Your task to perform on an android device: Open Google Chrome and click the shortcut for Amazon.com Image 0: 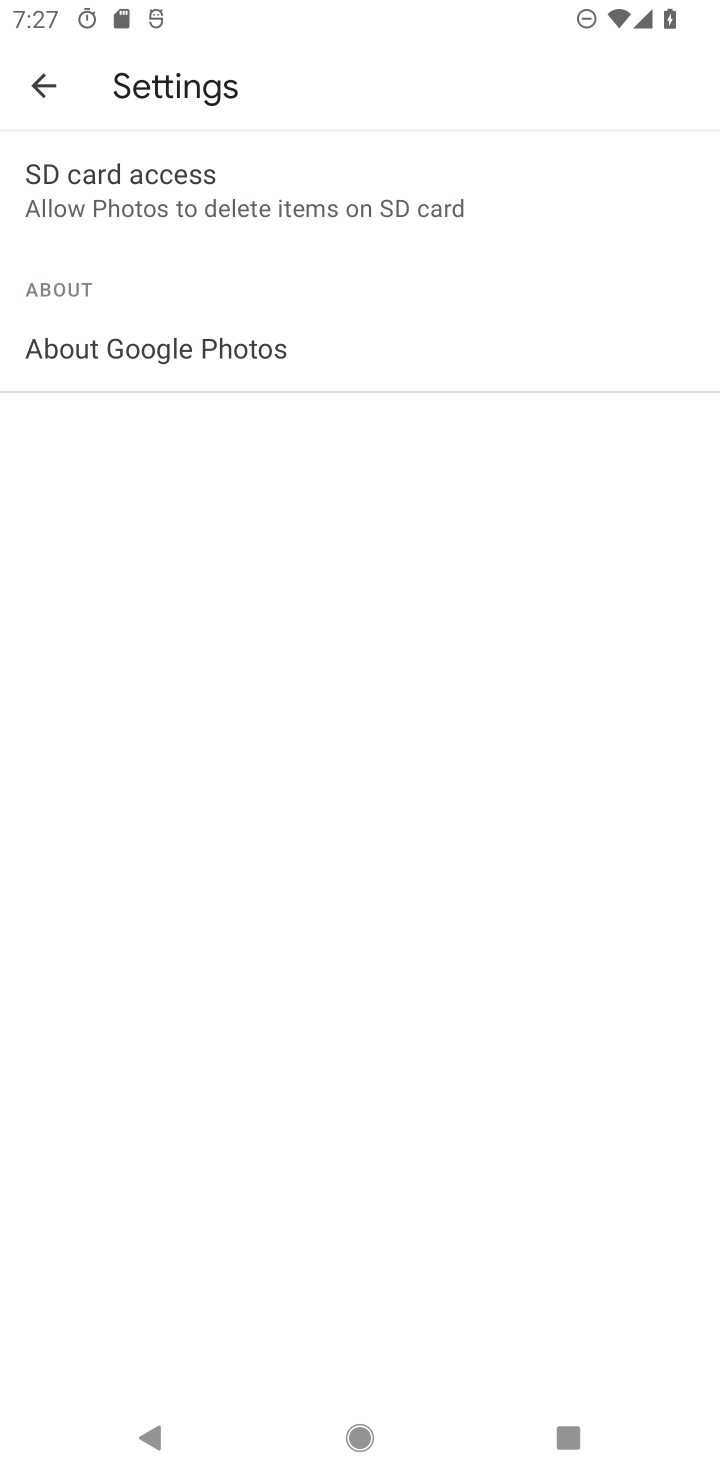
Step 0: press home button
Your task to perform on an android device: Open Google Chrome and click the shortcut for Amazon.com Image 1: 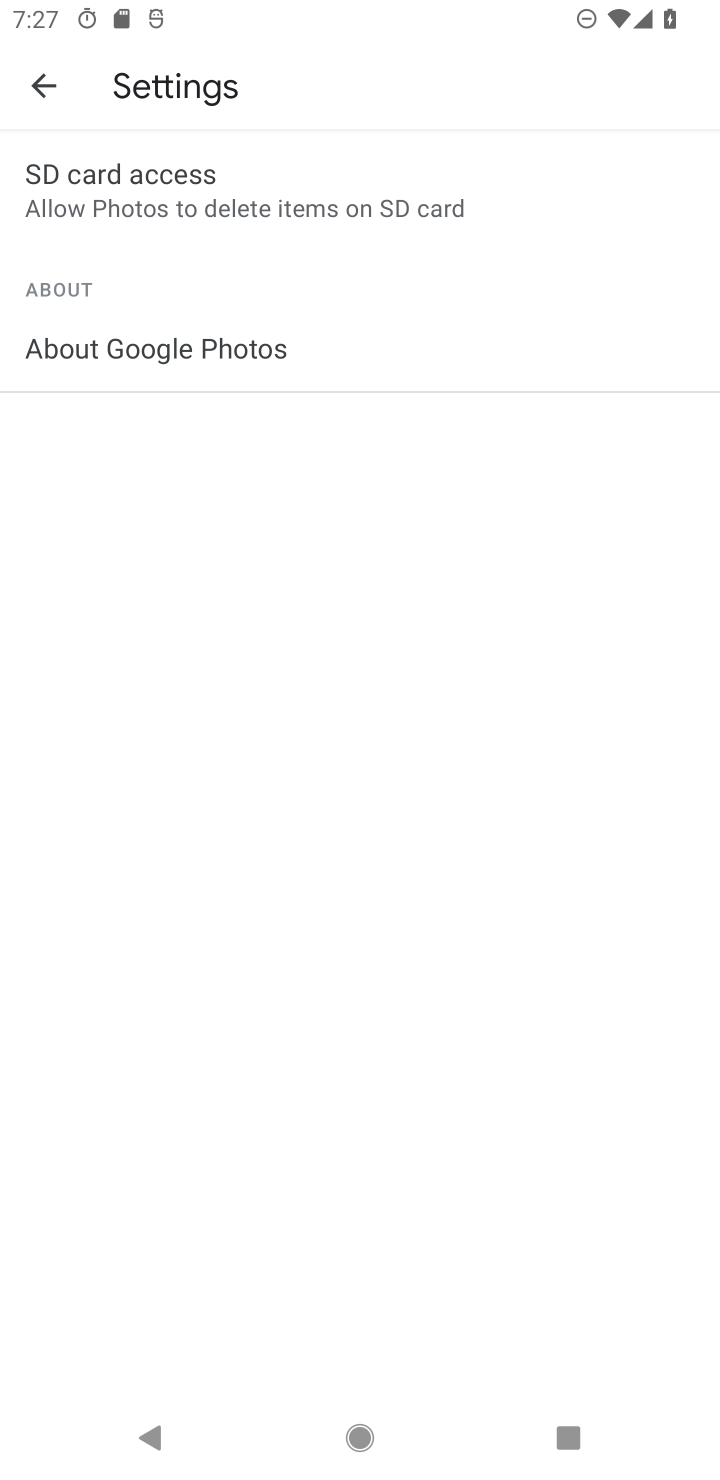
Step 1: drag from (459, 687) to (480, 224)
Your task to perform on an android device: Open Google Chrome and click the shortcut for Amazon.com Image 2: 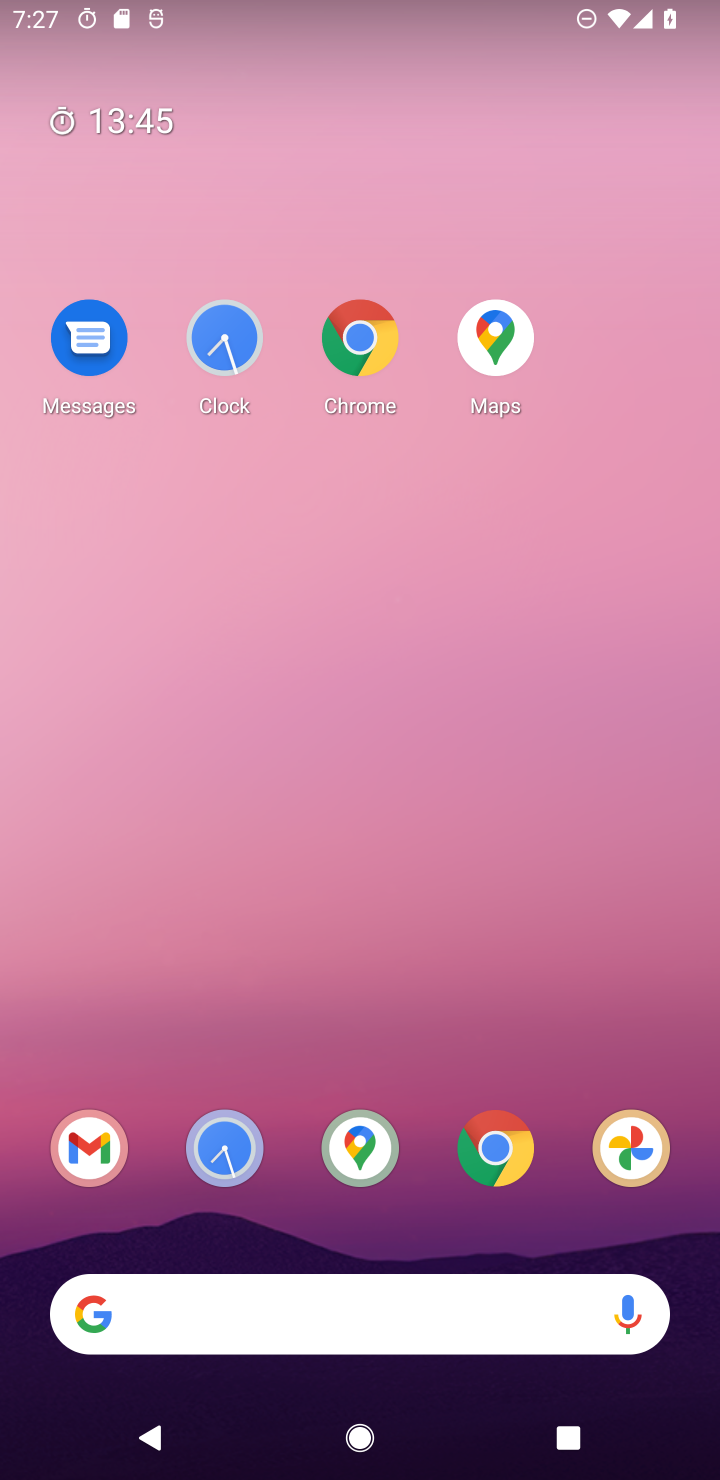
Step 2: drag from (416, 1092) to (445, 138)
Your task to perform on an android device: Open Google Chrome and click the shortcut for Amazon.com Image 3: 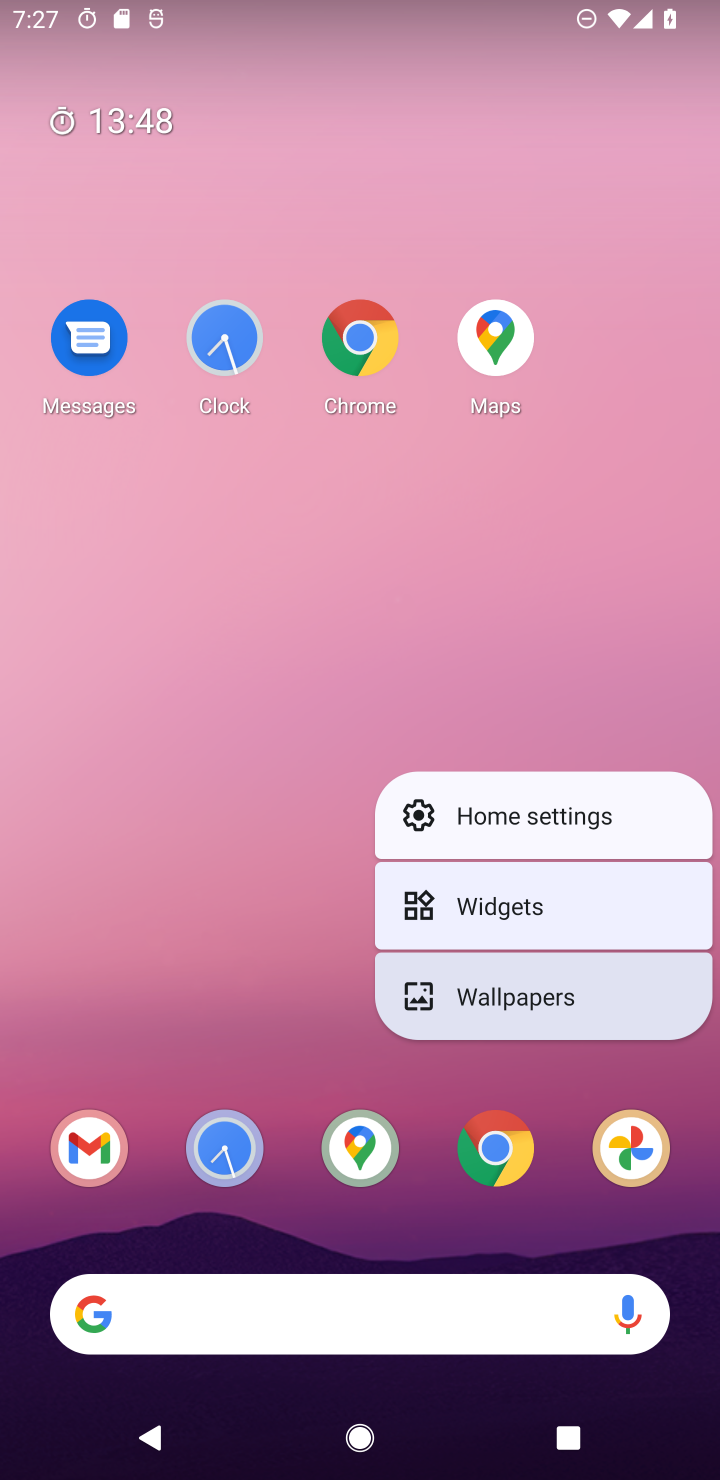
Step 3: click (498, 1144)
Your task to perform on an android device: Open Google Chrome and click the shortcut for Amazon.com Image 4: 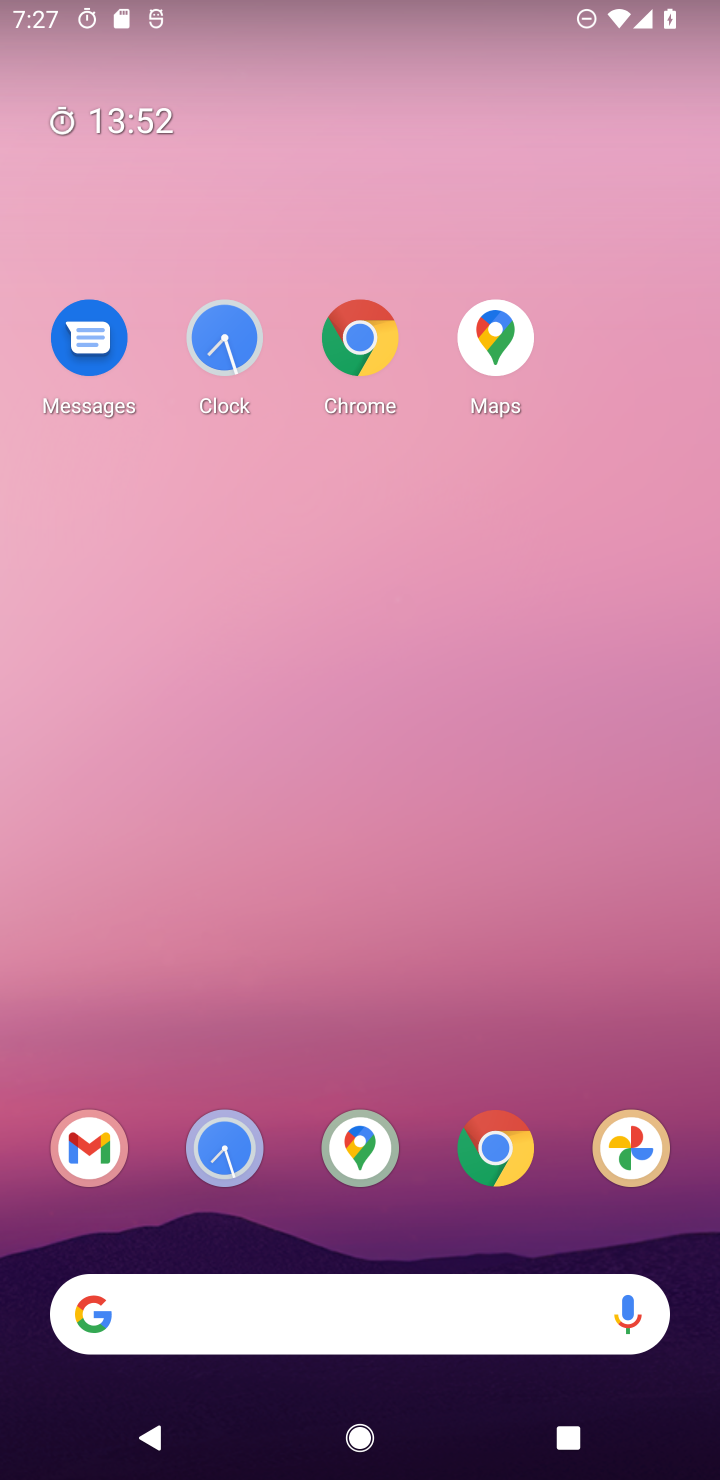
Step 4: click (488, 1131)
Your task to perform on an android device: Open Google Chrome and click the shortcut for Amazon.com Image 5: 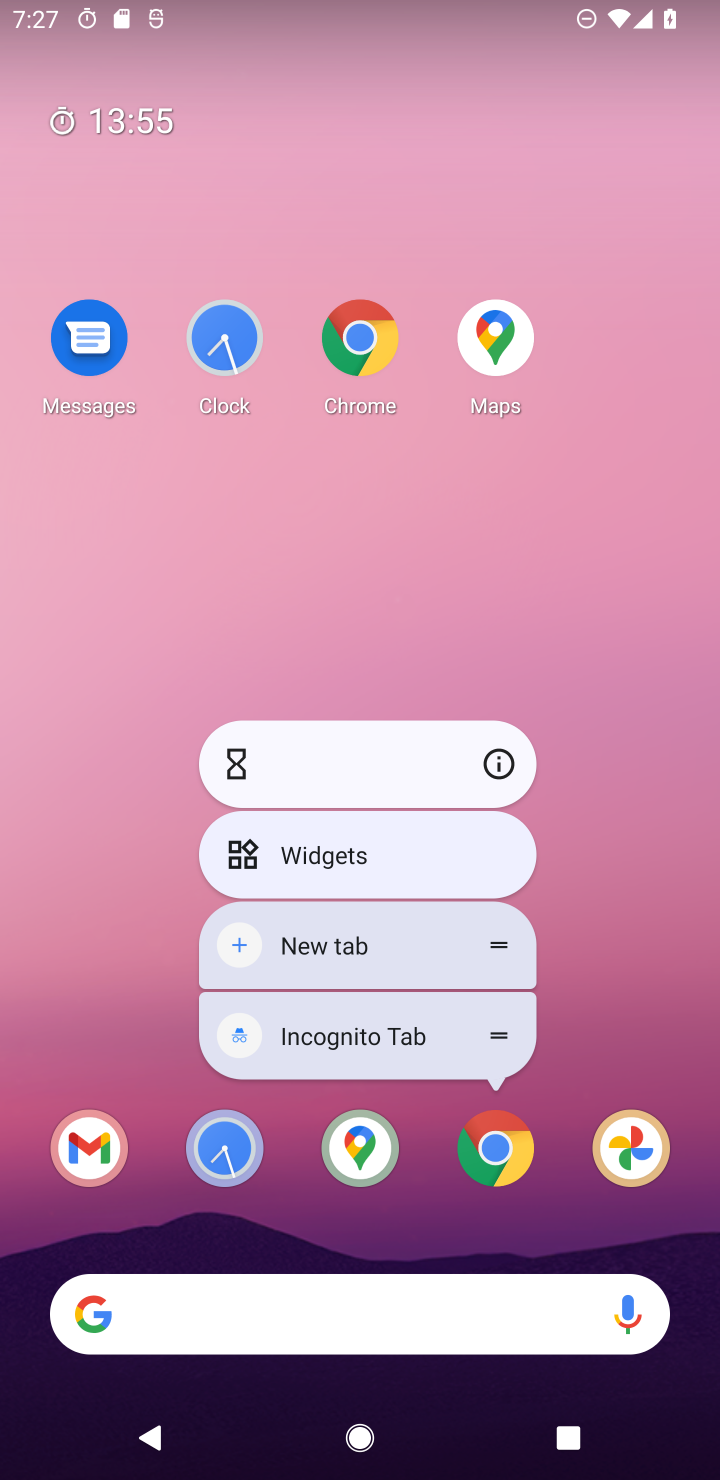
Step 5: click (482, 742)
Your task to perform on an android device: Open Google Chrome and click the shortcut for Amazon.com Image 6: 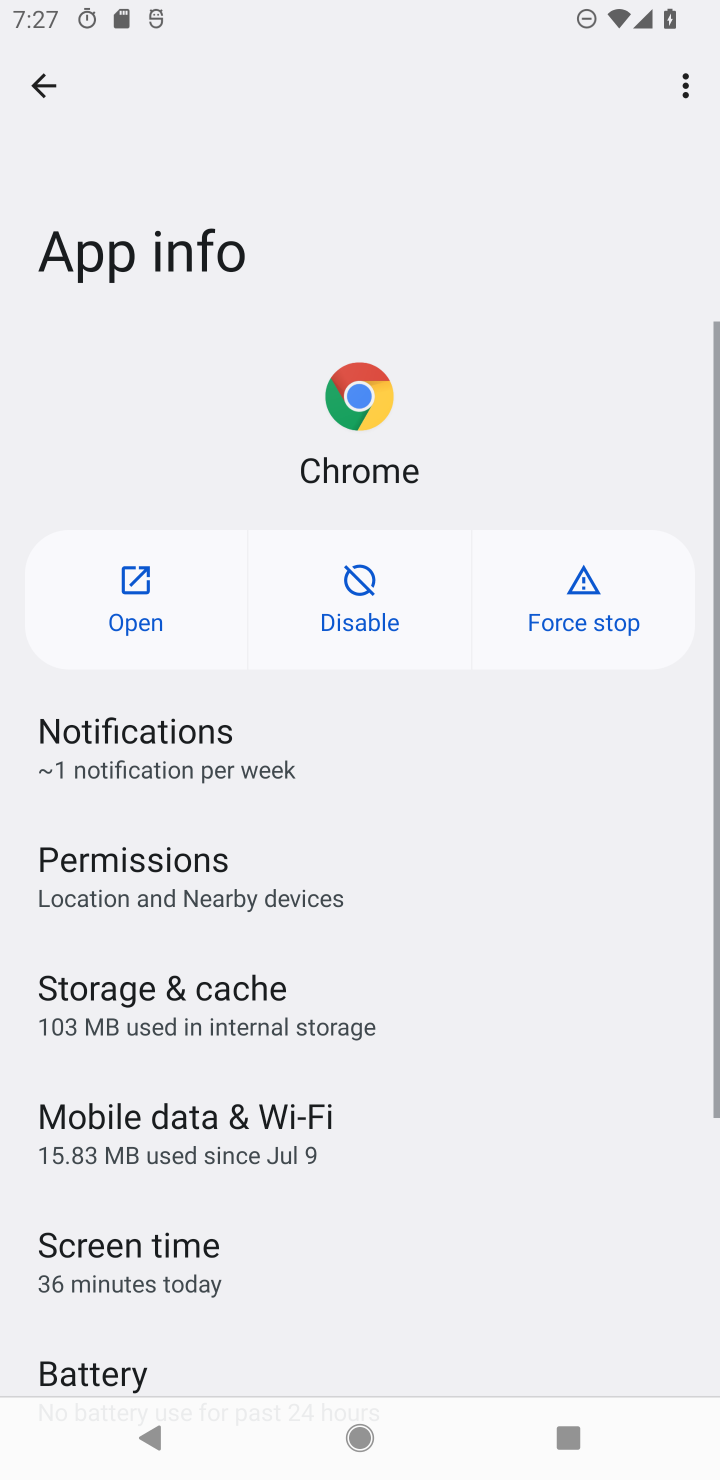
Step 6: click (137, 569)
Your task to perform on an android device: Open Google Chrome and click the shortcut for Amazon.com Image 7: 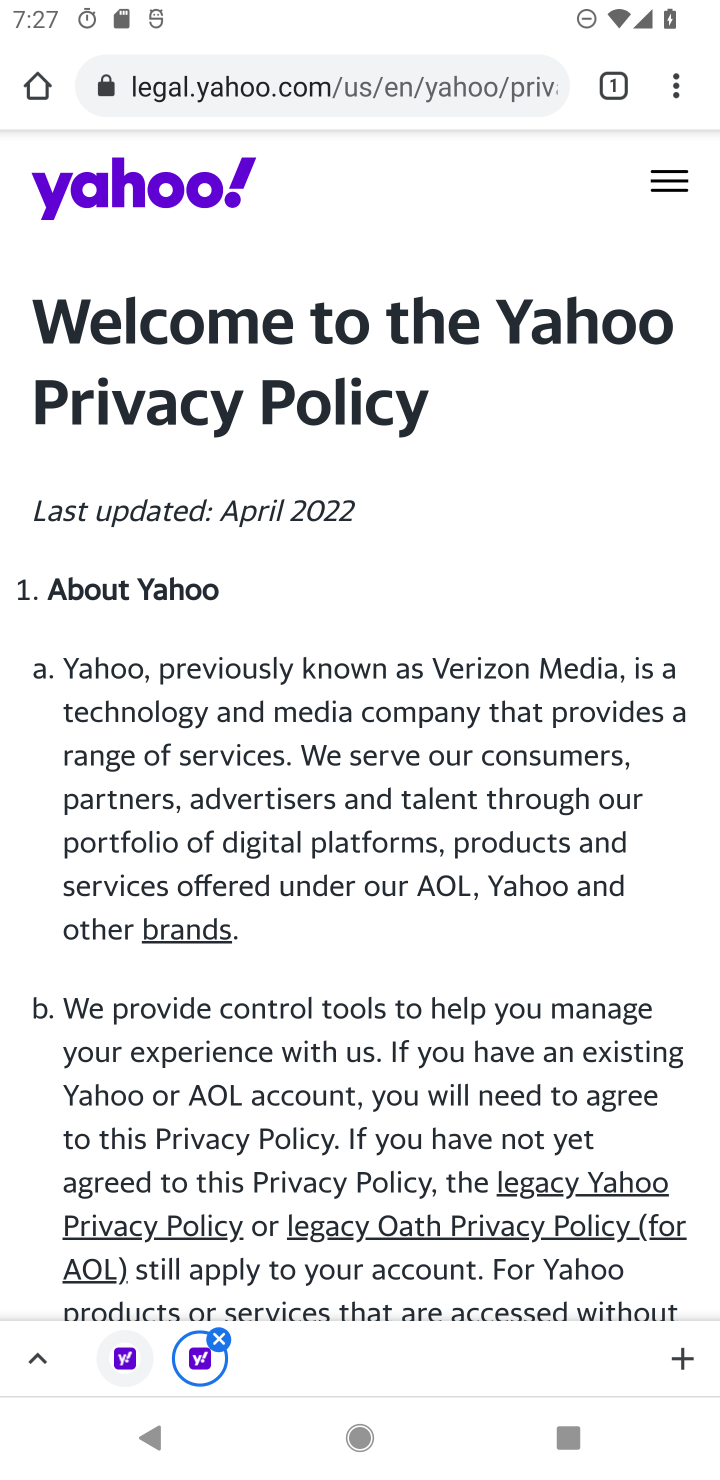
Step 7: click (620, 89)
Your task to perform on an android device: Open Google Chrome and click the shortcut for Amazon.com Image 8: 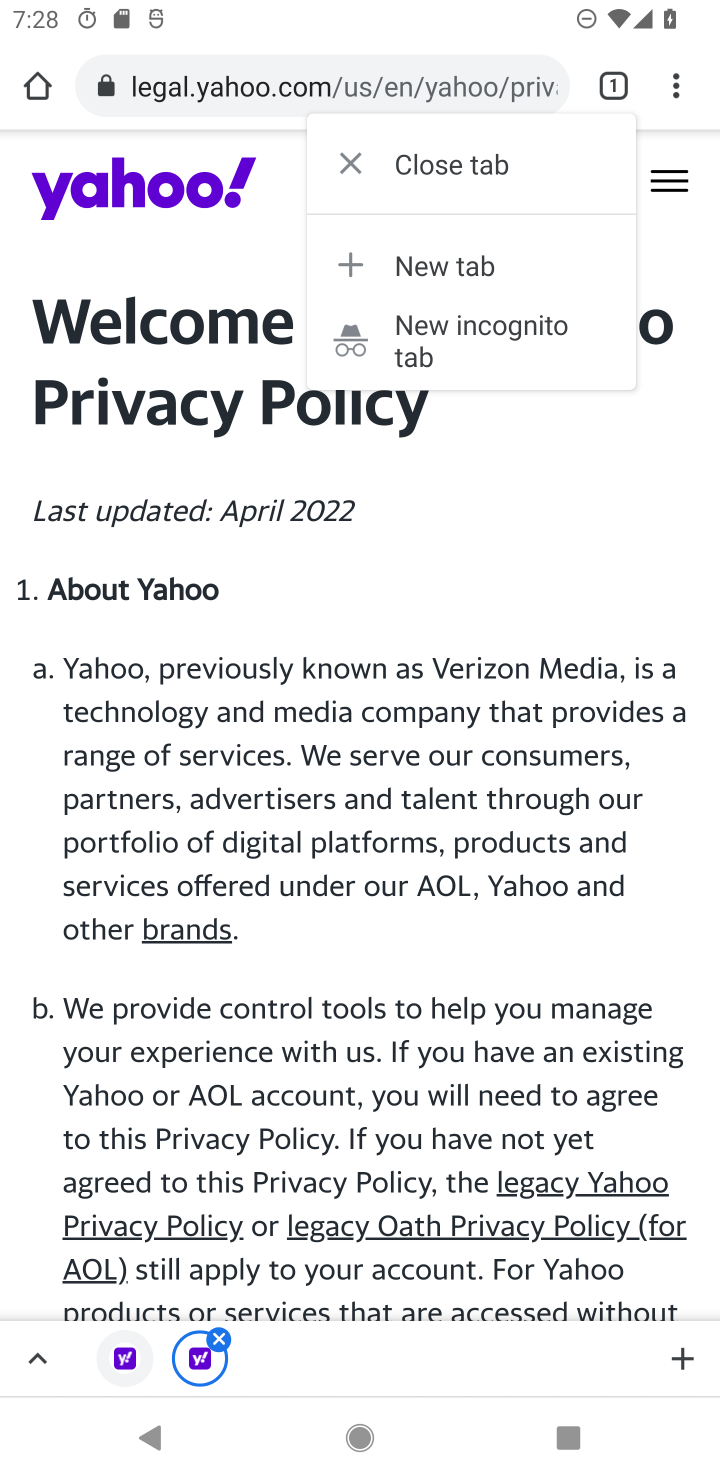
Step 8: click (492, 264)
Your task to perform on an android device: Open Google Chrome and click the shortcut for Amazon.com Image 9: 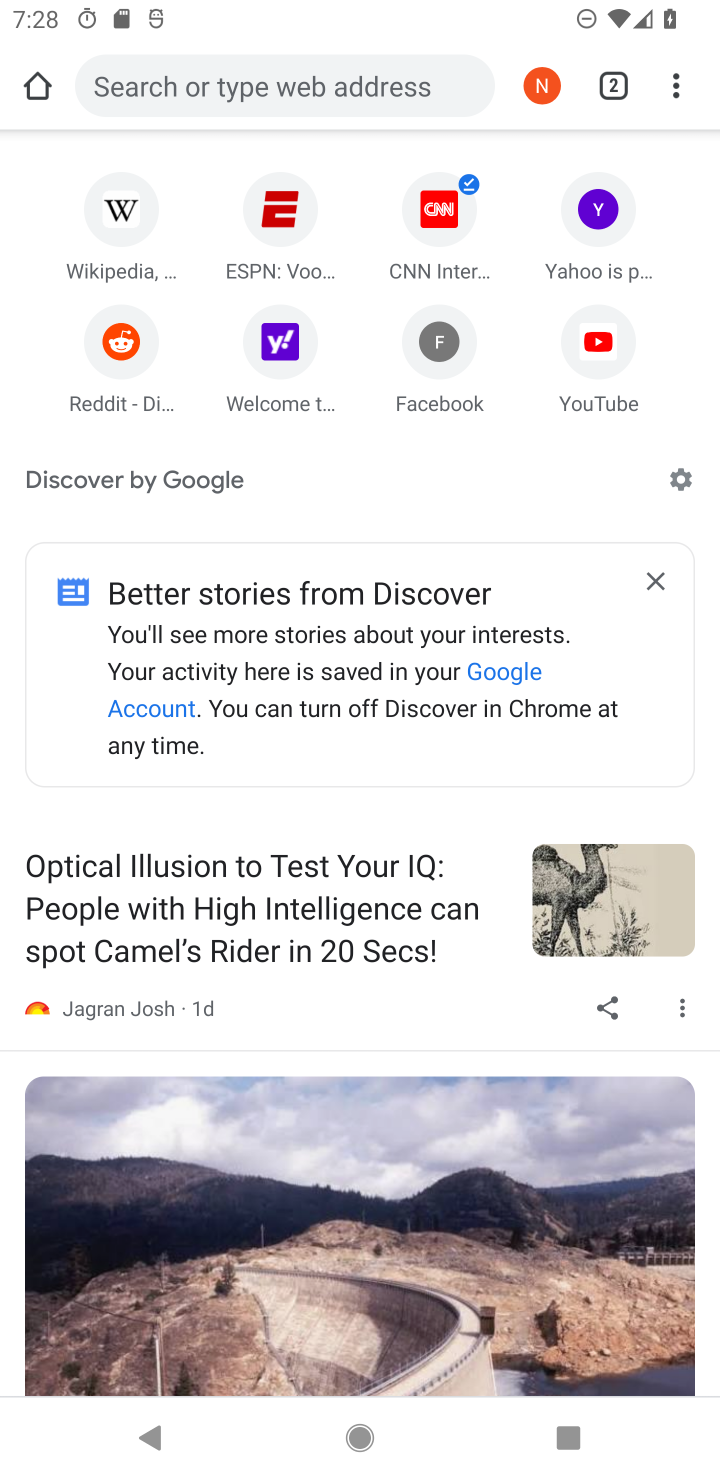
Step 9: drag from (380, 905) to (386, 260)
Your task to perform on an android device: Open Google Chrome and click the shortcut for Amazon.com Image 10: 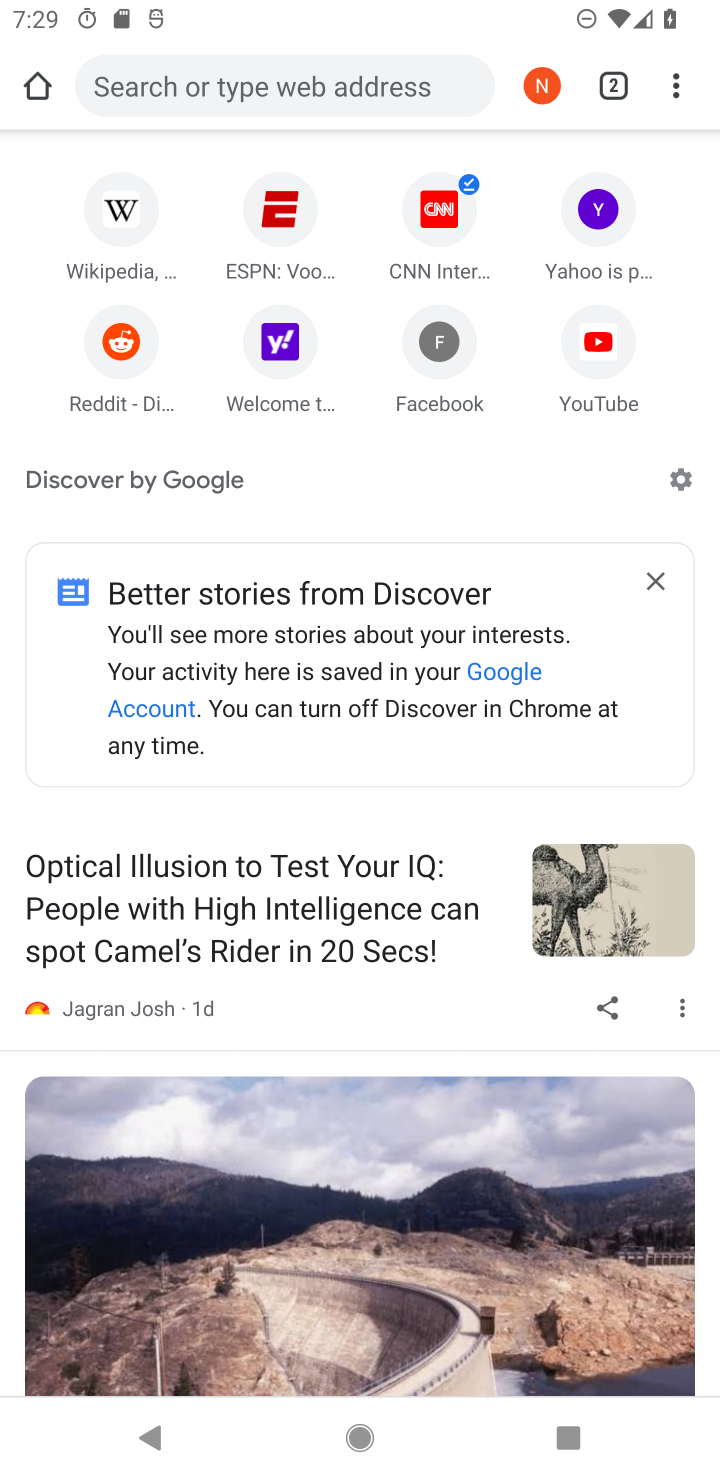
Step 10: drag from (377, 698) to (411, 337)
Your task to perform on an android device: Open Google Chrome and click the shortcut for Amazon.com Image 11: 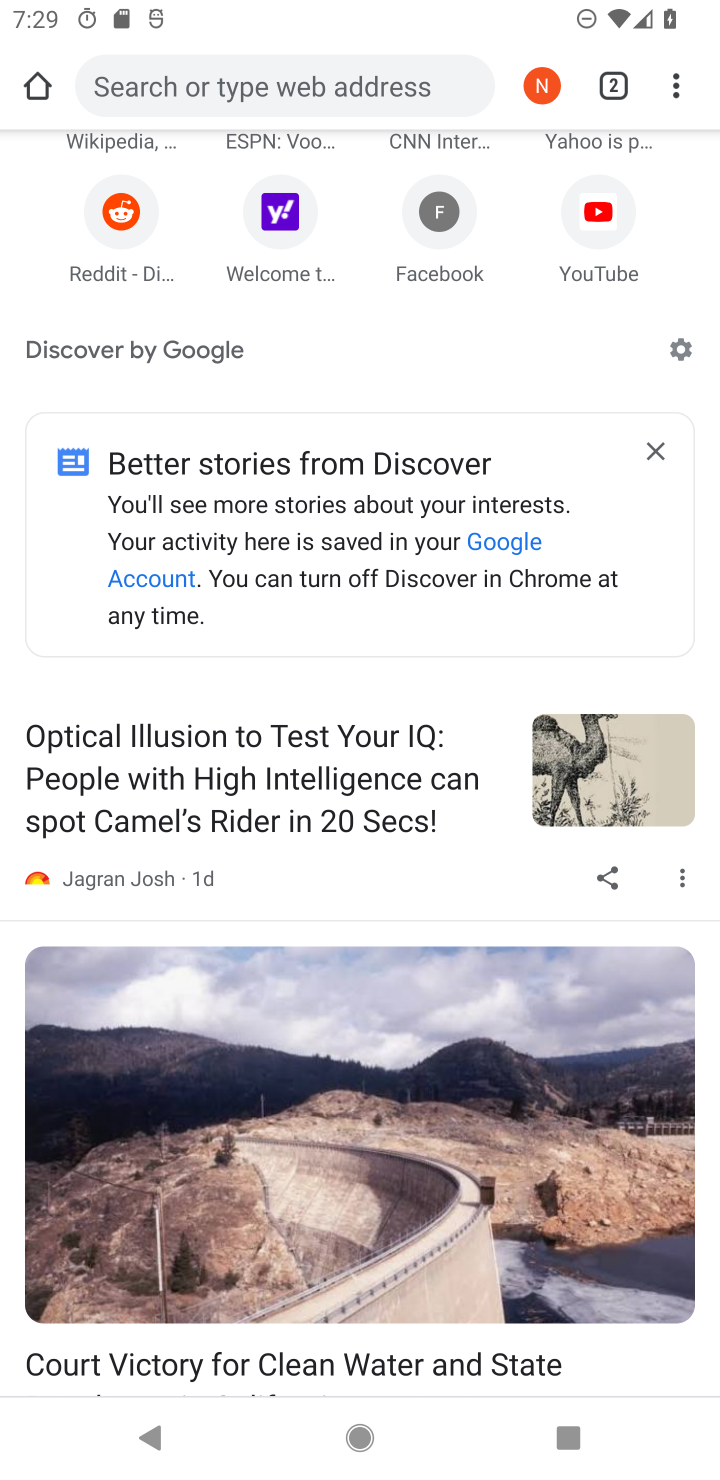
Step 11: drag from (442, 434) to (442, 265)
Your task to perform on an android device: Open Google Chrome and click the shortcut for Amazon.com Image 12: 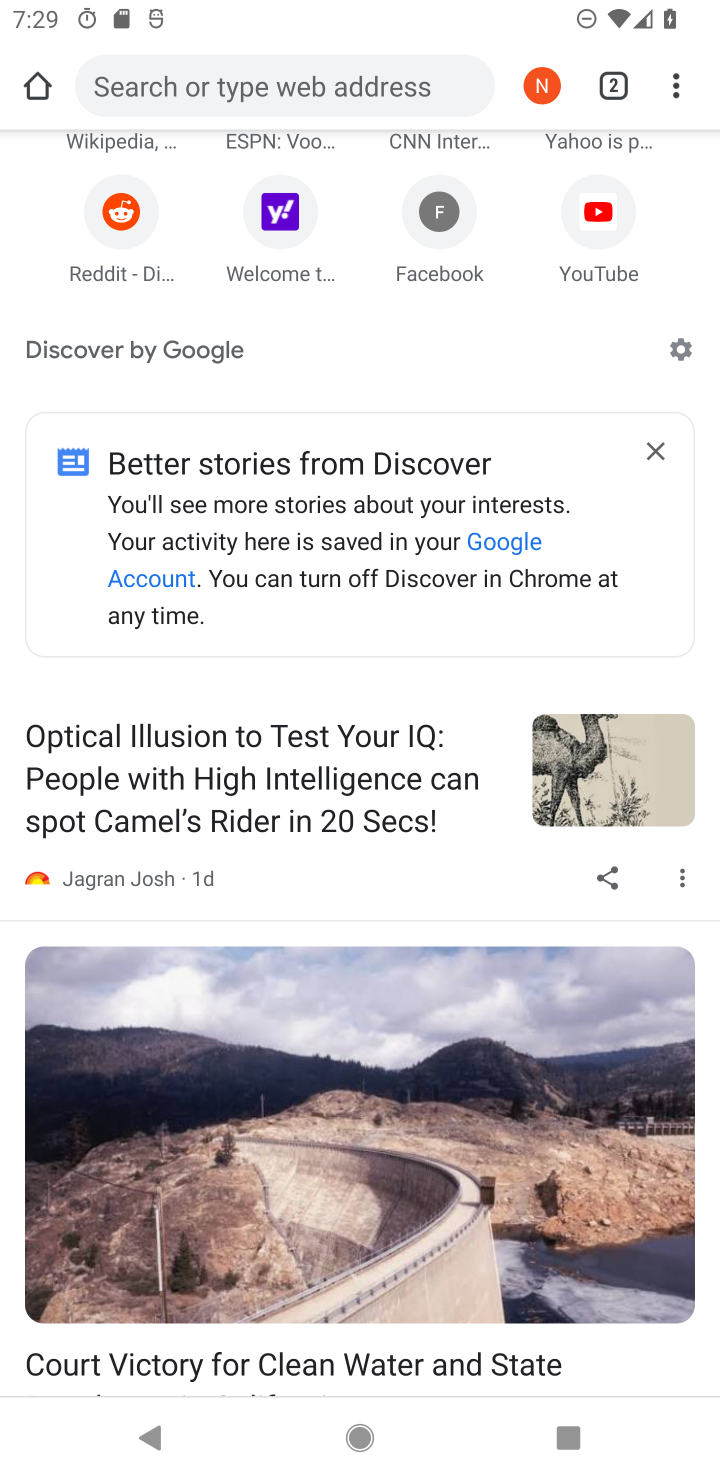
Step 12: drag from (376, 741) to (376, 358)
Your task to perform on an android device: Open Google Chrome and click the shortcut for Amazon.com Image 13: 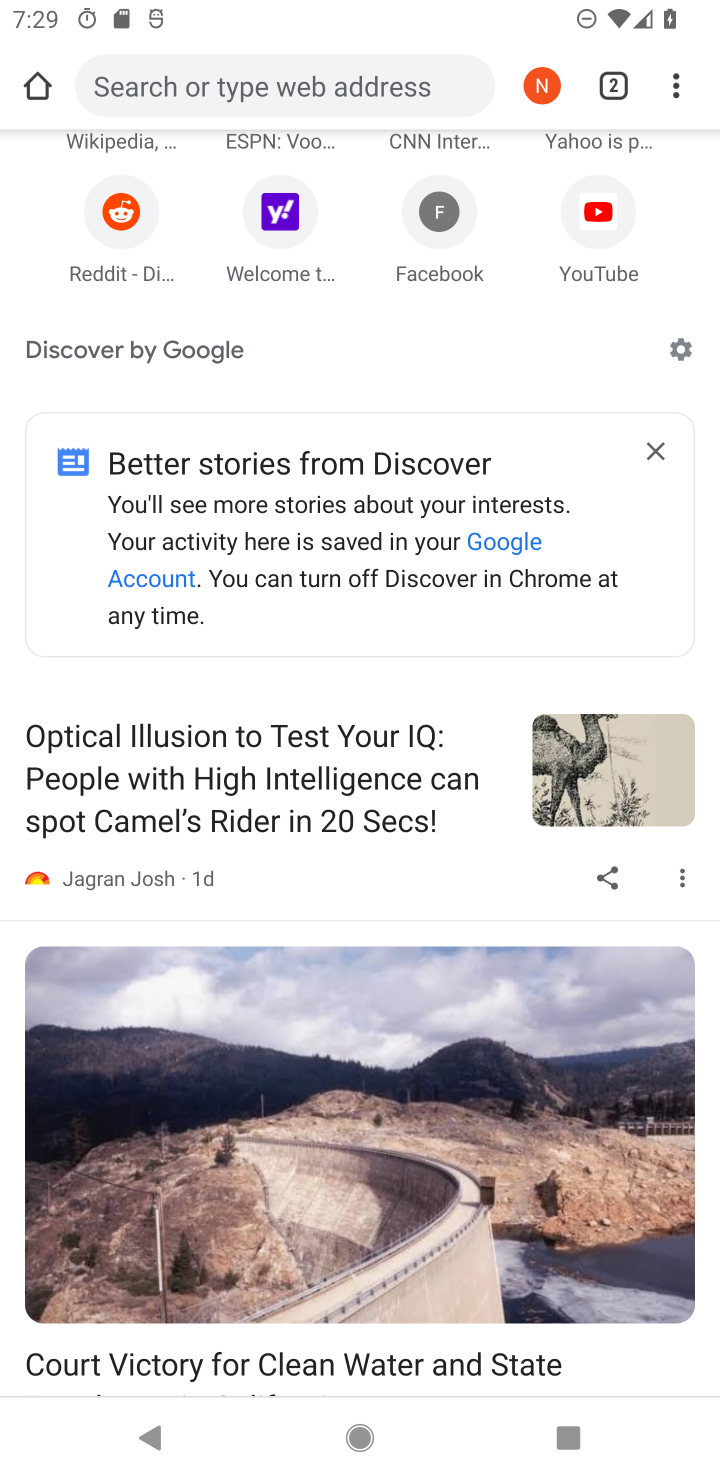
Step 13: click (557, 1449)
Your task to perform on an android device: Open Google Chrome and click the shortcut for Amazon.com Image 14: 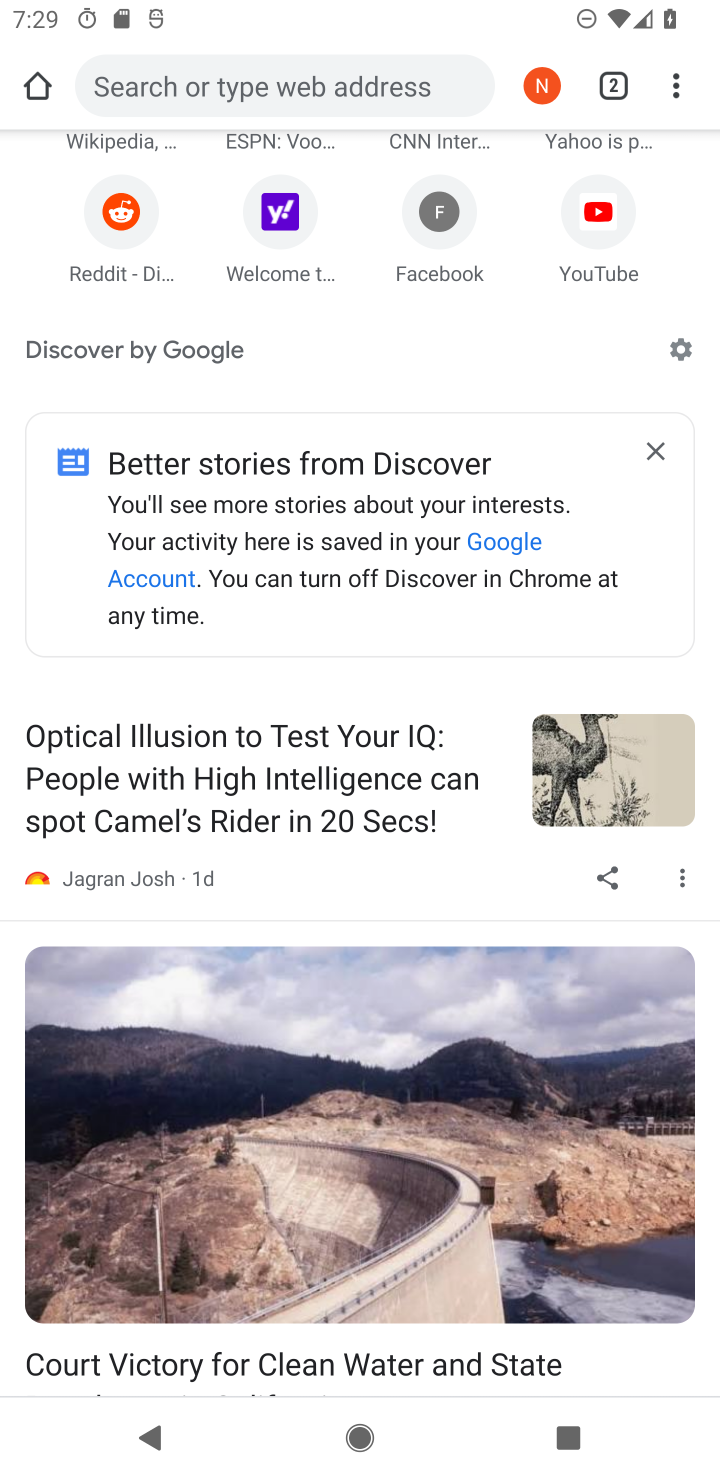
Step 14: click (171, 90)
Your task to perform on an android device: Open Google Chrome and click the shortcut for Amazon.com Image 15: 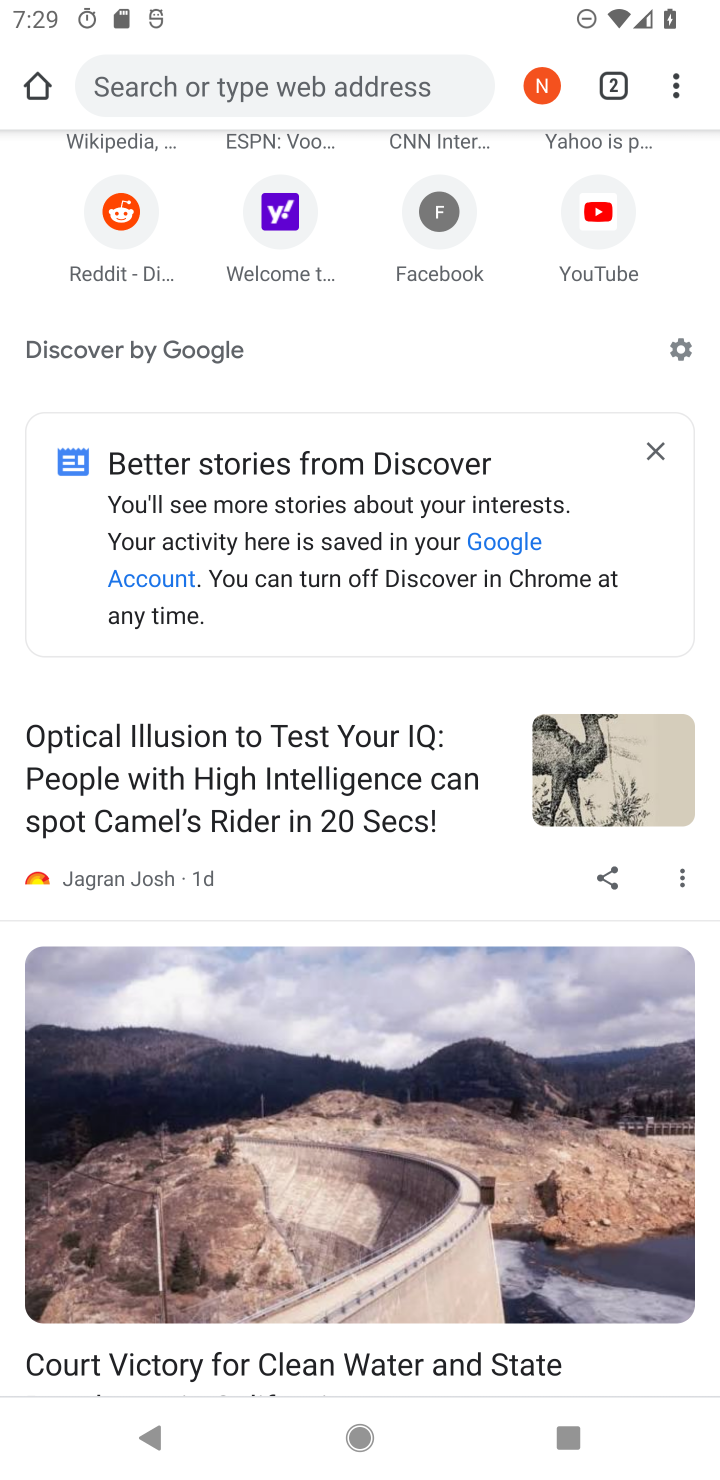
Step 15: drag from (415, 727) to (516, 1286)
Your task to perform on an android device: Open Google Chrome and click the shortcut for Amazon.com Image 16: 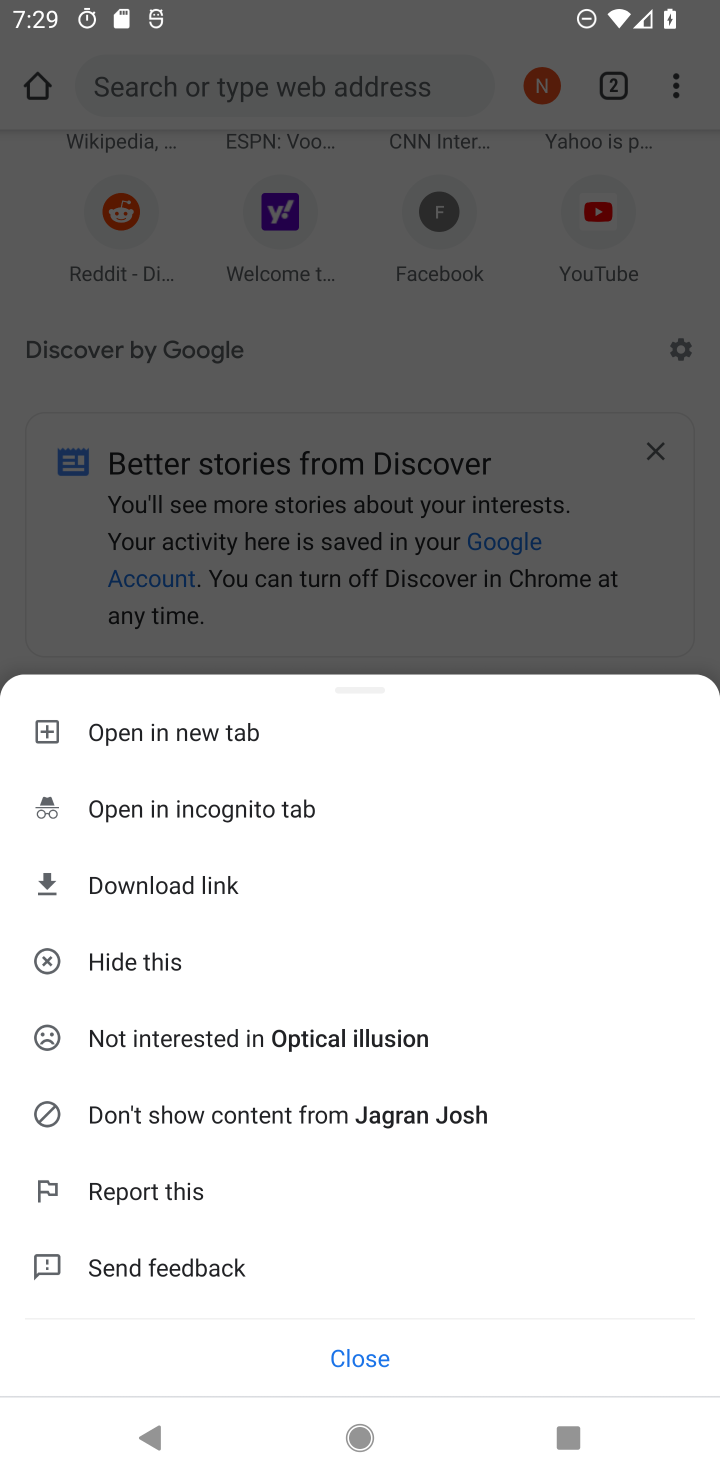
Step 16: drag from (378, 425) to (305, 1254)
Your task to perform on an android device: Open Google Chrome and click the shortcut for Amazon.com Image 17: 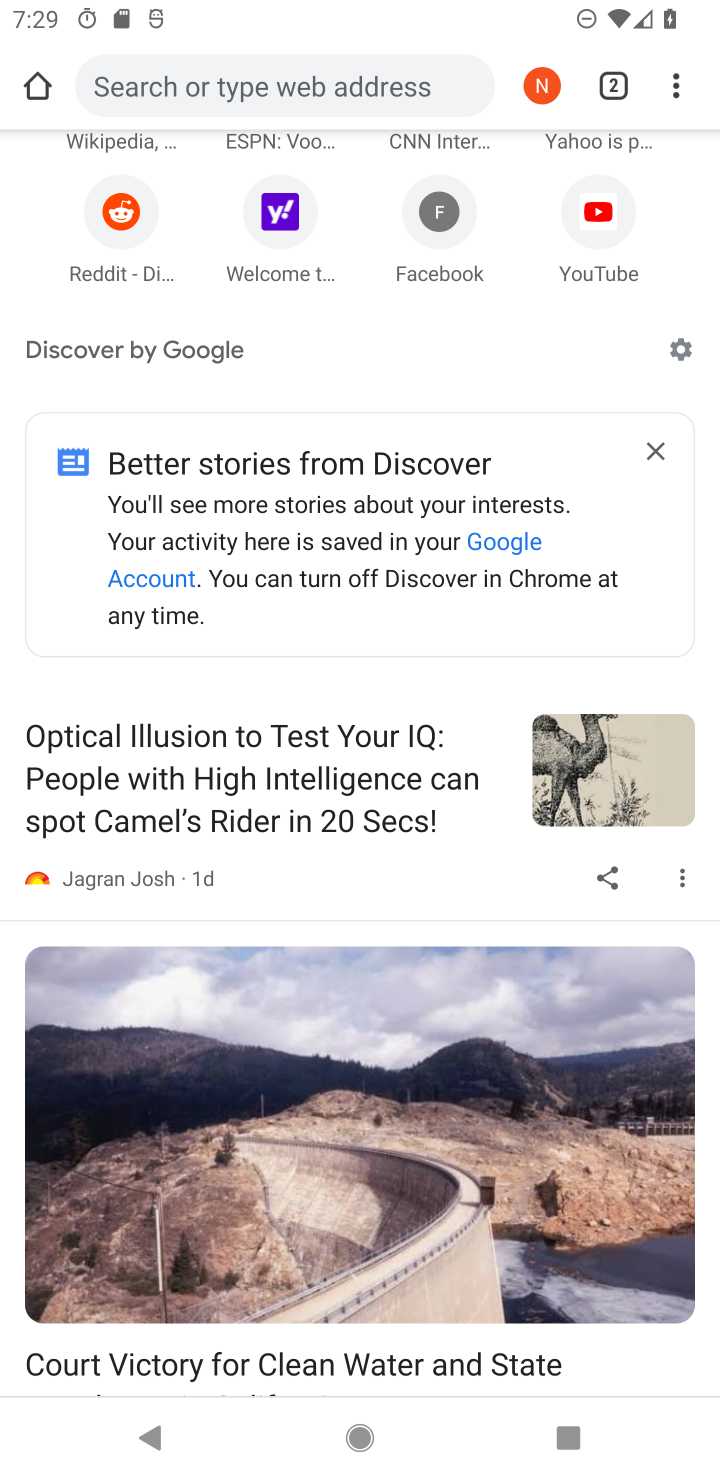
Step 17: click (350, 1365)
Your task to perform on an android device: Open Google Chrome and click the shortcut for Amazon.com Image 18: 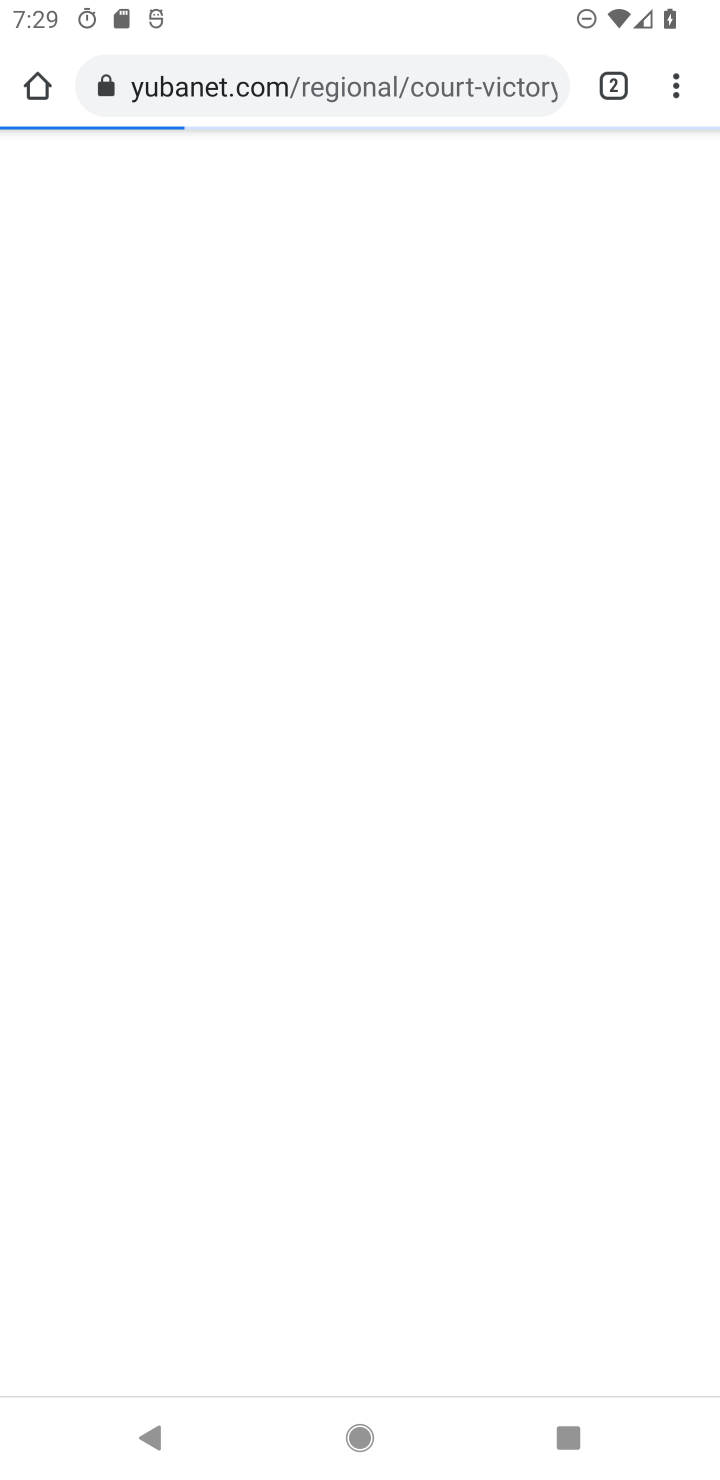
Step 18: drag from (452, 1139) to (551, 1445)
Your task to perform on an android device: Open Google Chrome and click the shortcut for Amazon.com Image 19: 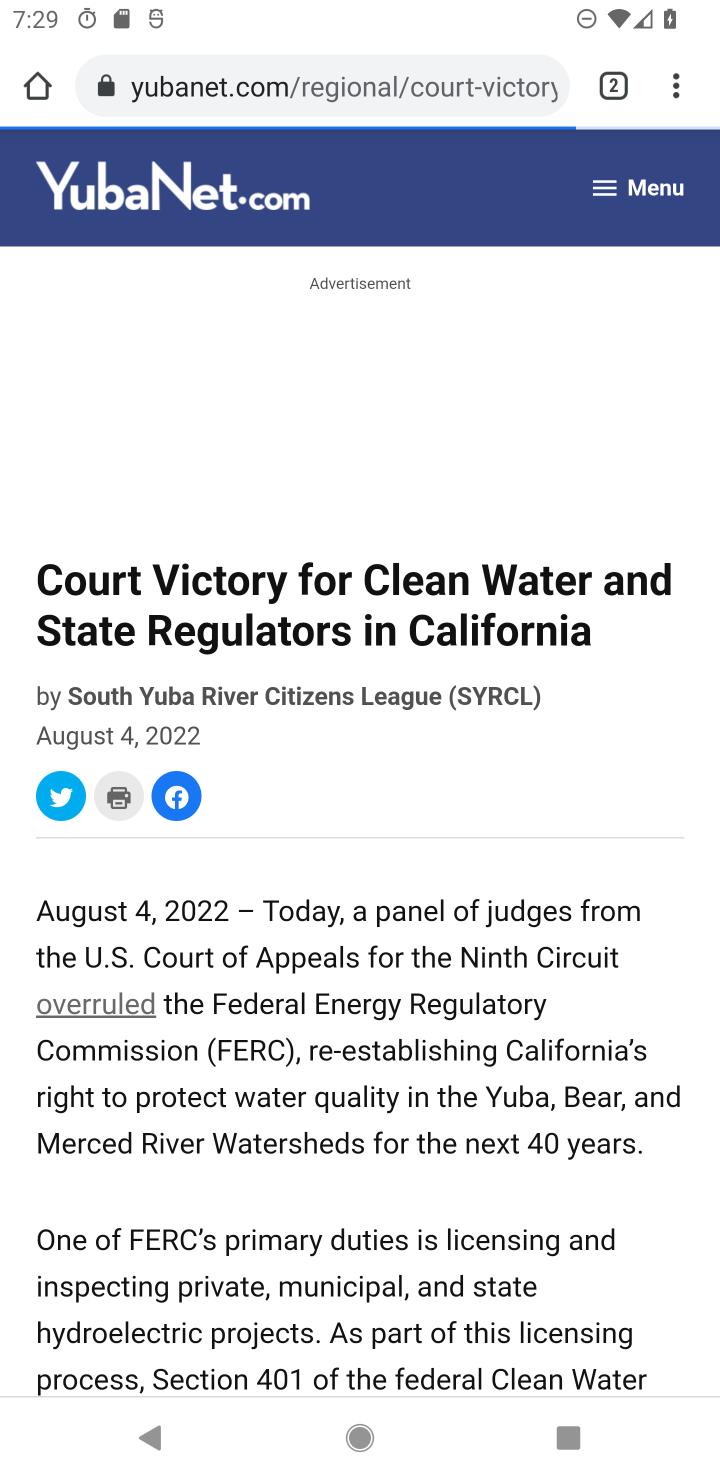
Step 19: drag from (332, 327) to (487, 1135)
Your task to perform on an android device: Open Google Chrome and click the shortcut for Amazon.com Image 20: 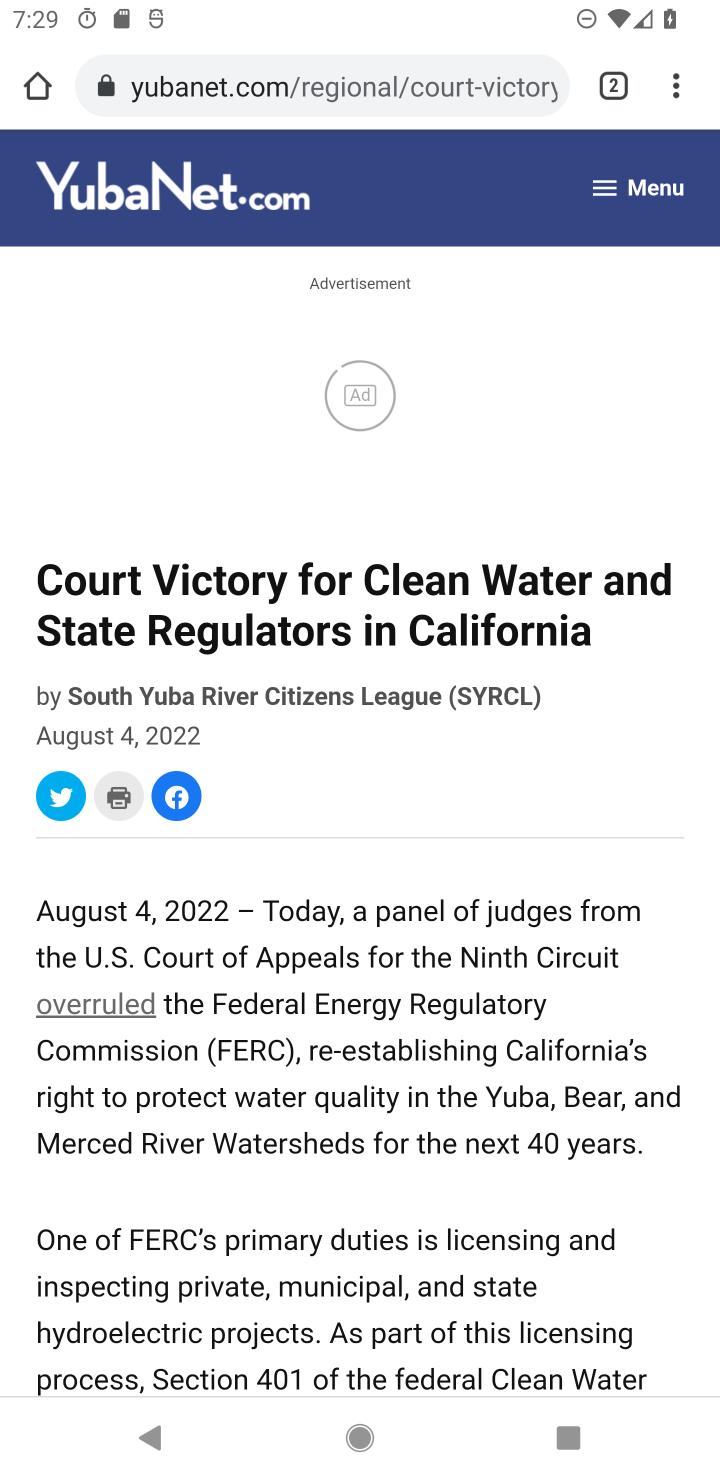
Step 20: click (262, 94)
Your task to perform on an android device: Open Google Chrome and click the shortcut for Amazon.com Image 21: 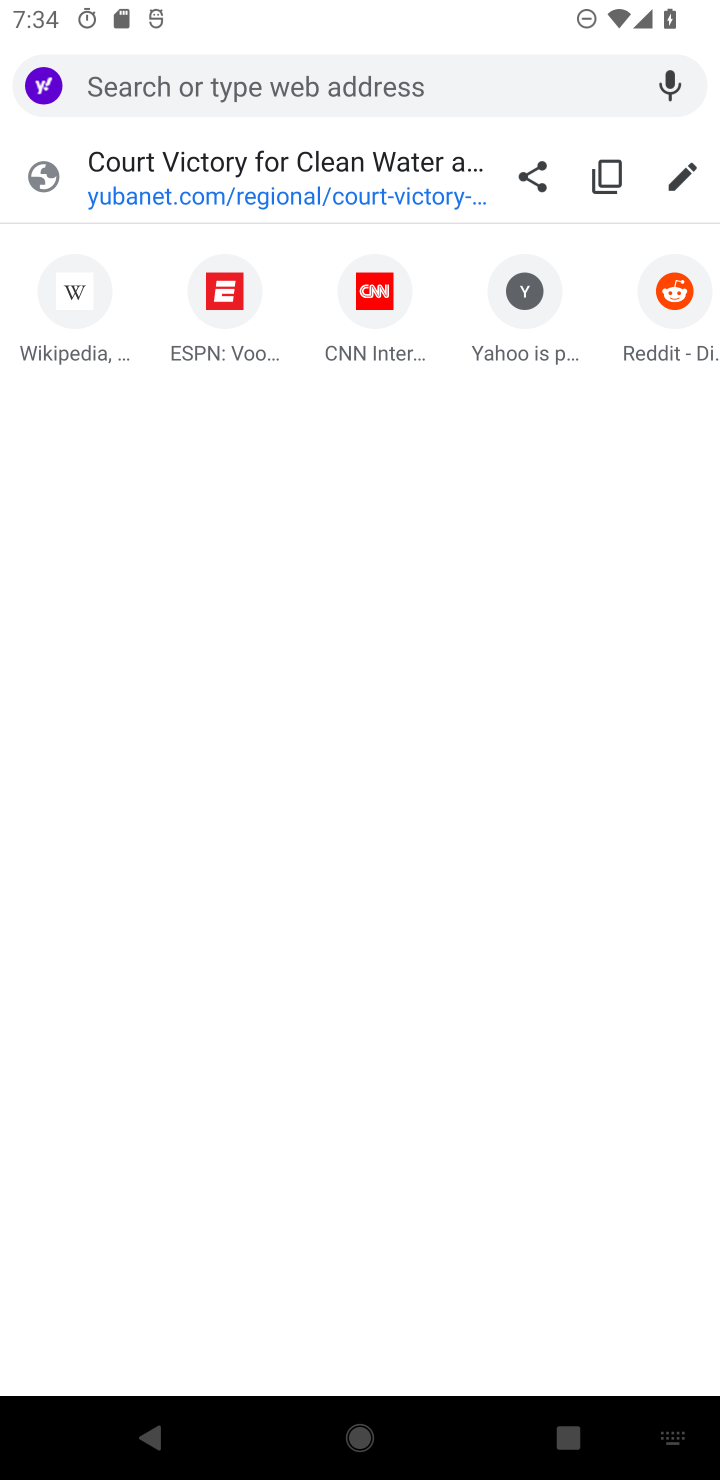
Step 21: click (392, 604)
Your task to perform on an android device: Open Google Chrome and click the shortcut for Amazon.com Image 22: 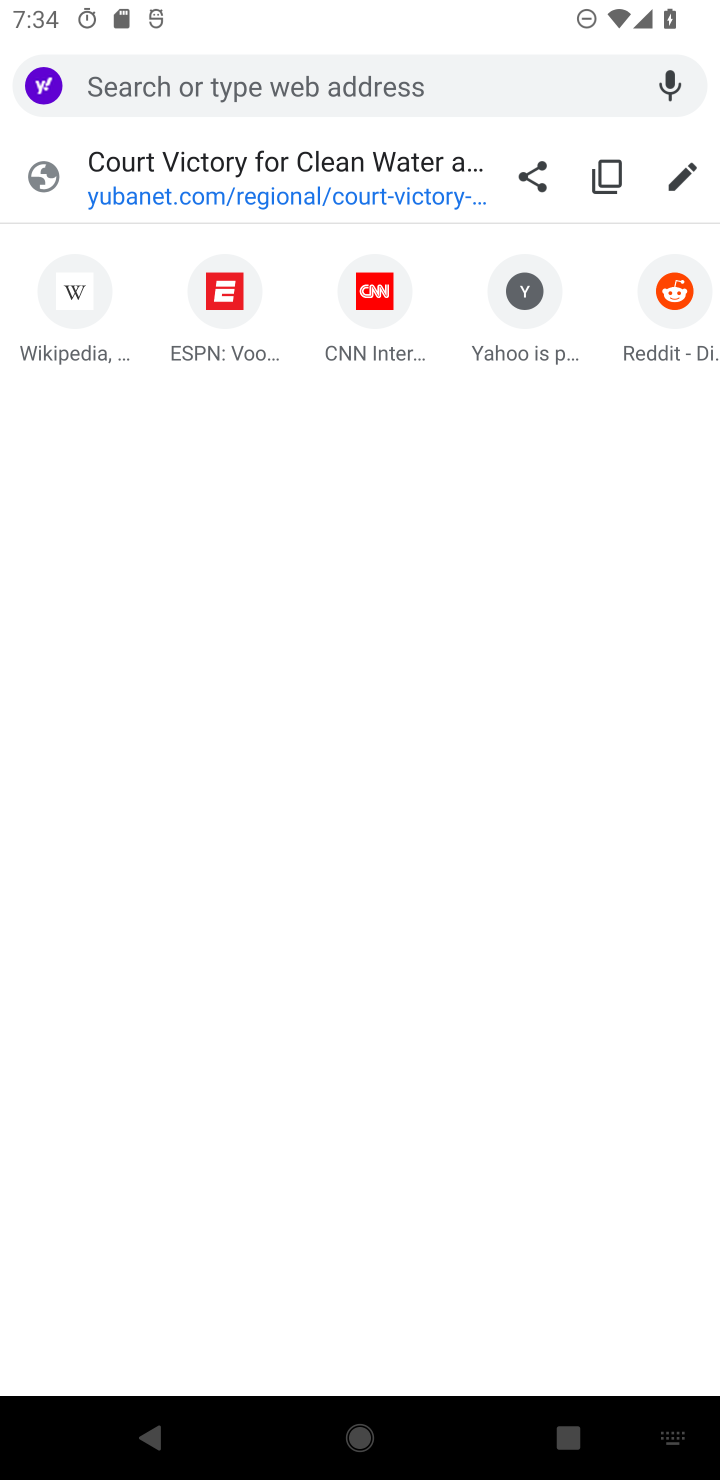
Step 22: click (391, 922)
Your task to perform on an android device: Open Google Chrome and click the shortcut for Amazon.com Image 23: 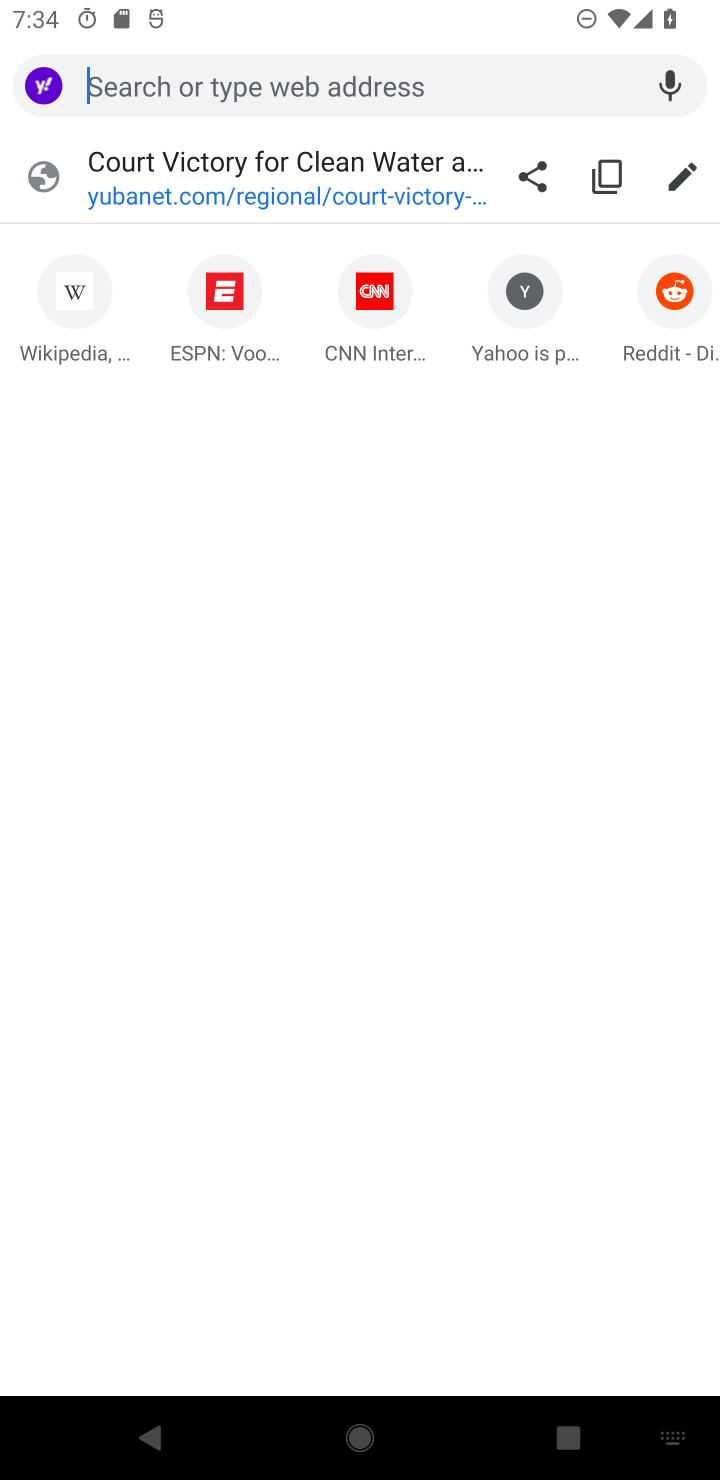
Step 23: press home button
Your task to perform on an android device: Open Google Chrome and click the shortcut for Amazon.com Image 24: 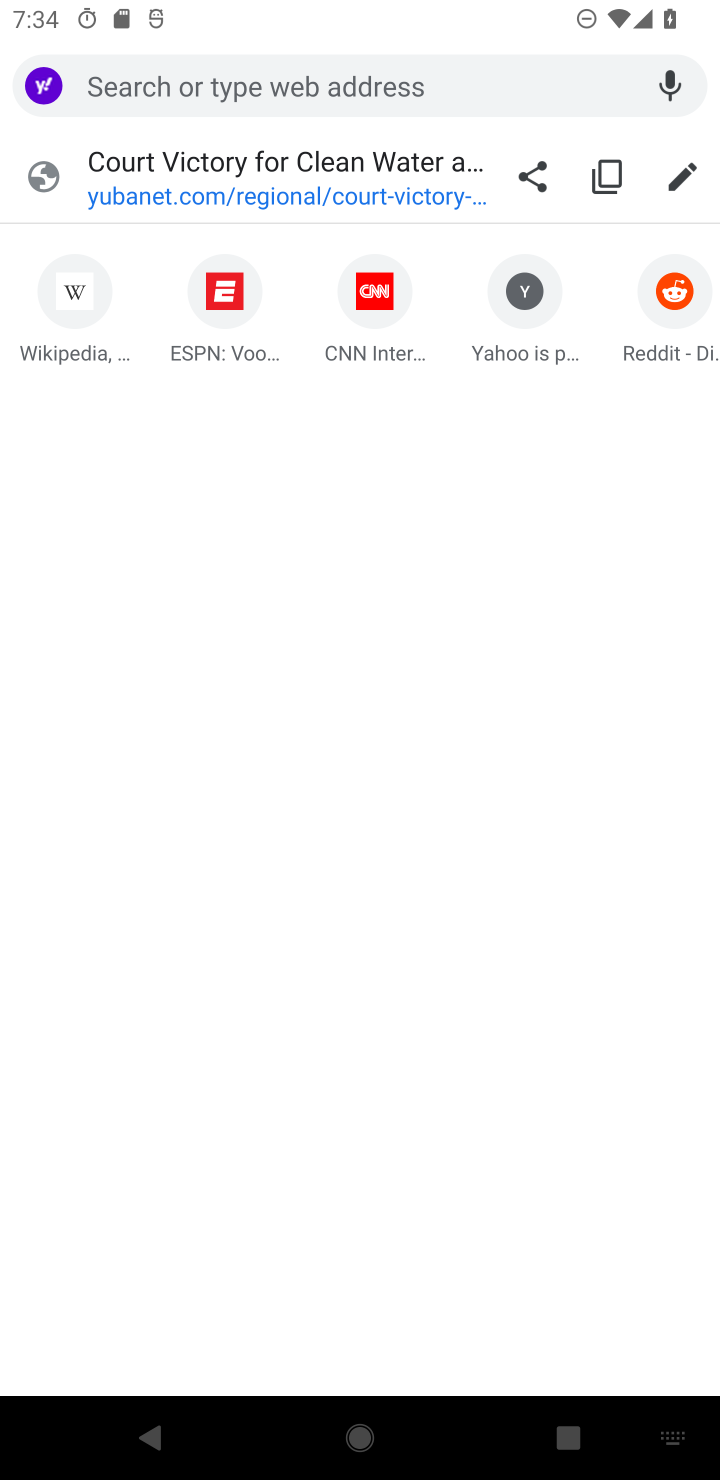
Step 24: drag from (346, 886) to (469, 278)
Your task to perform on an android device: Open Google Chrome and click the shortcut for Amazon.com Image 25: 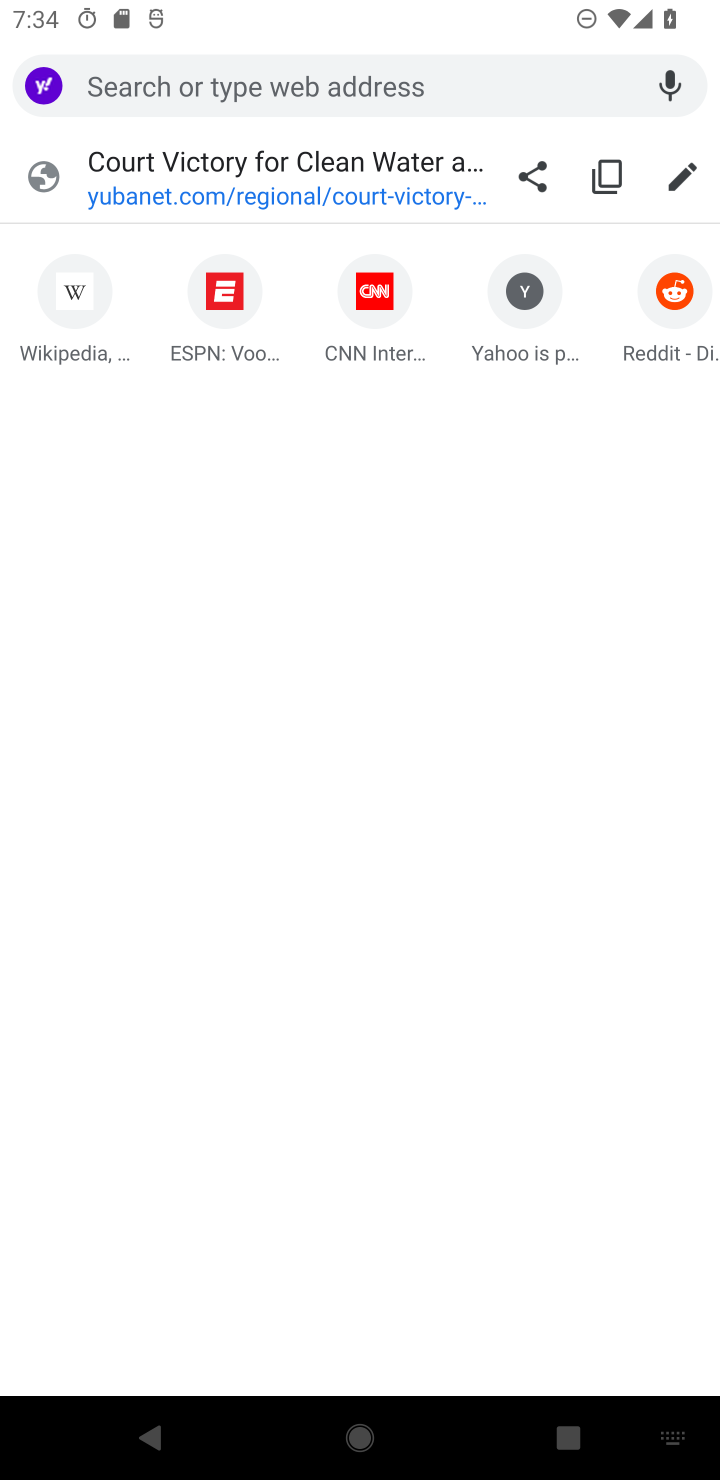
Step 25: press home button
Your task to perform on an android device: Open Google Chrome and click the shortcut for Amazon.com Image 26: 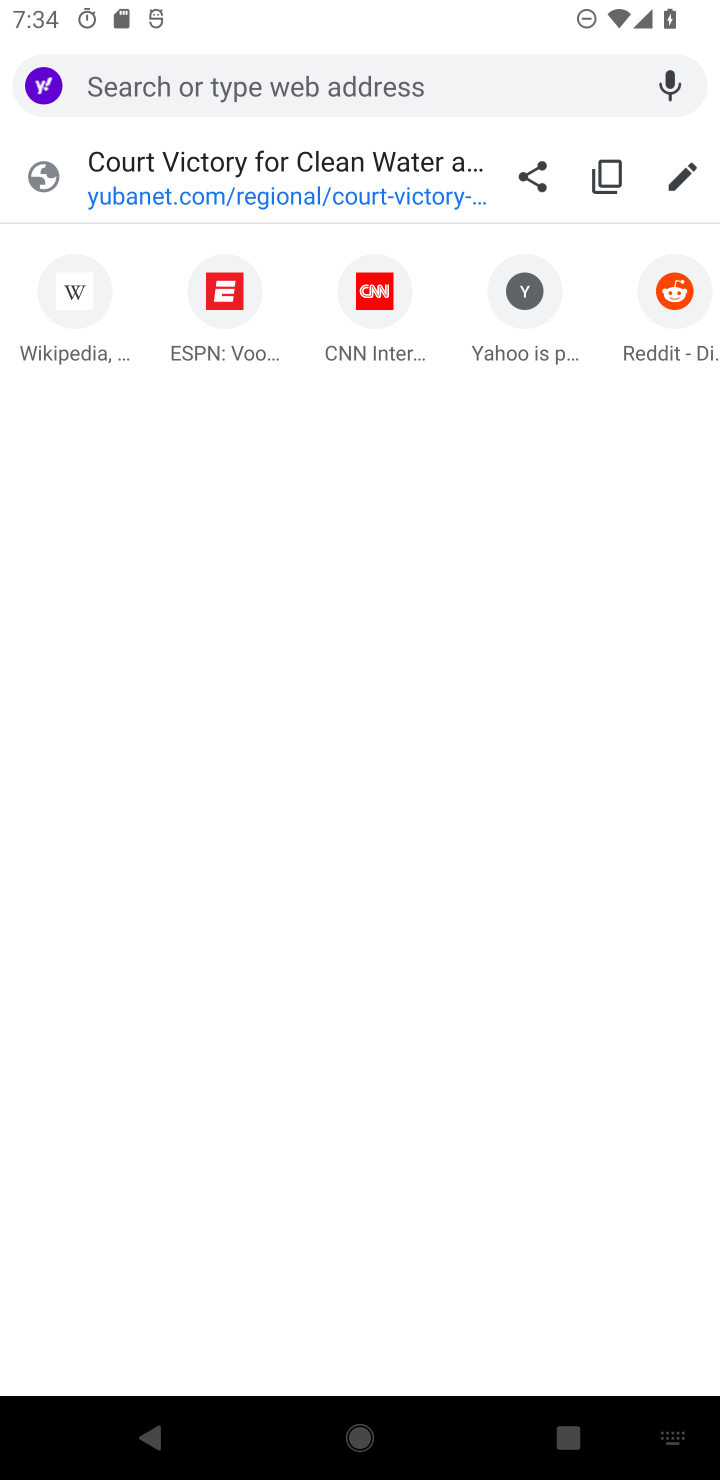
Step 26: click (539, 187)
Your task to perform on an android device: Open Google Chrome and click the shortcut for Amazon.com Image 27: 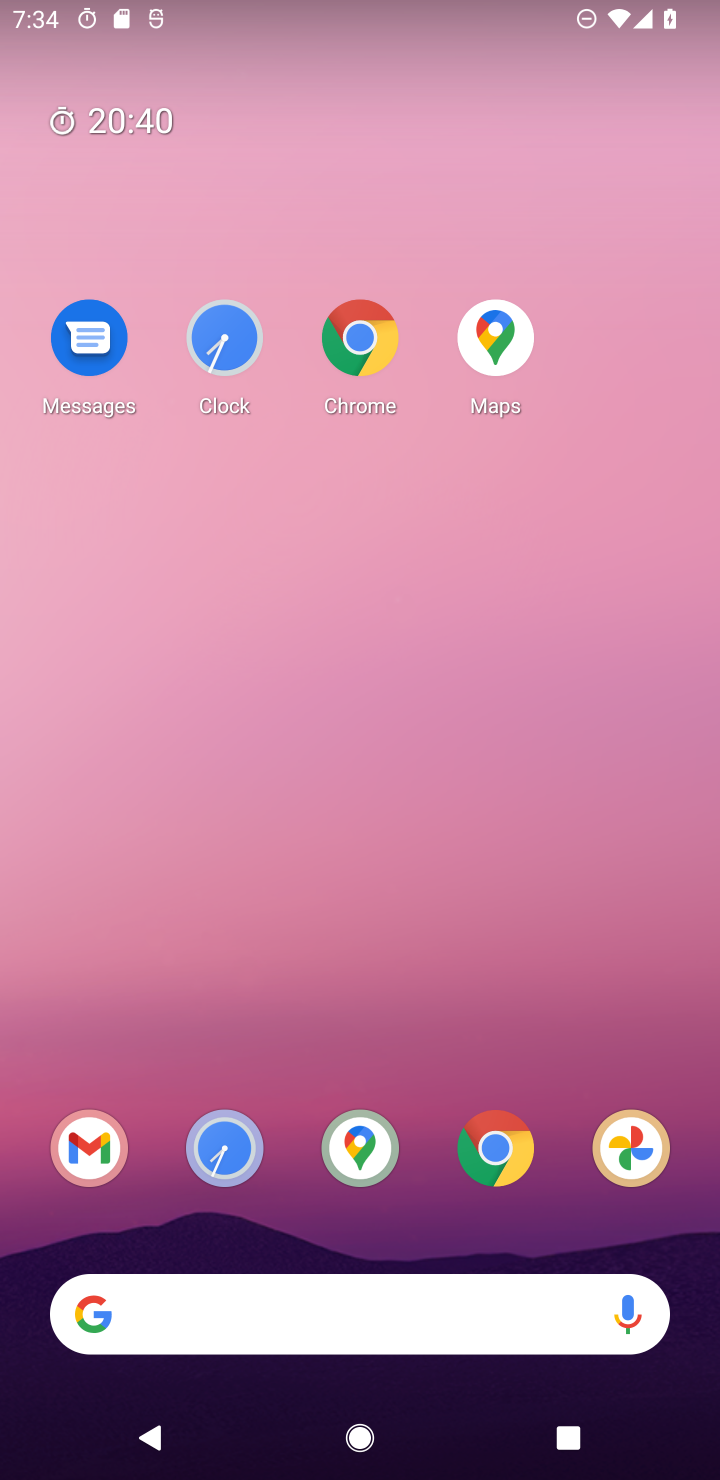
Step 27: drag from (329, 818) to (444, 324)
Your task to perform on an android device: Open Google Chrome and click the shortcut for Amazon.com Image 28: 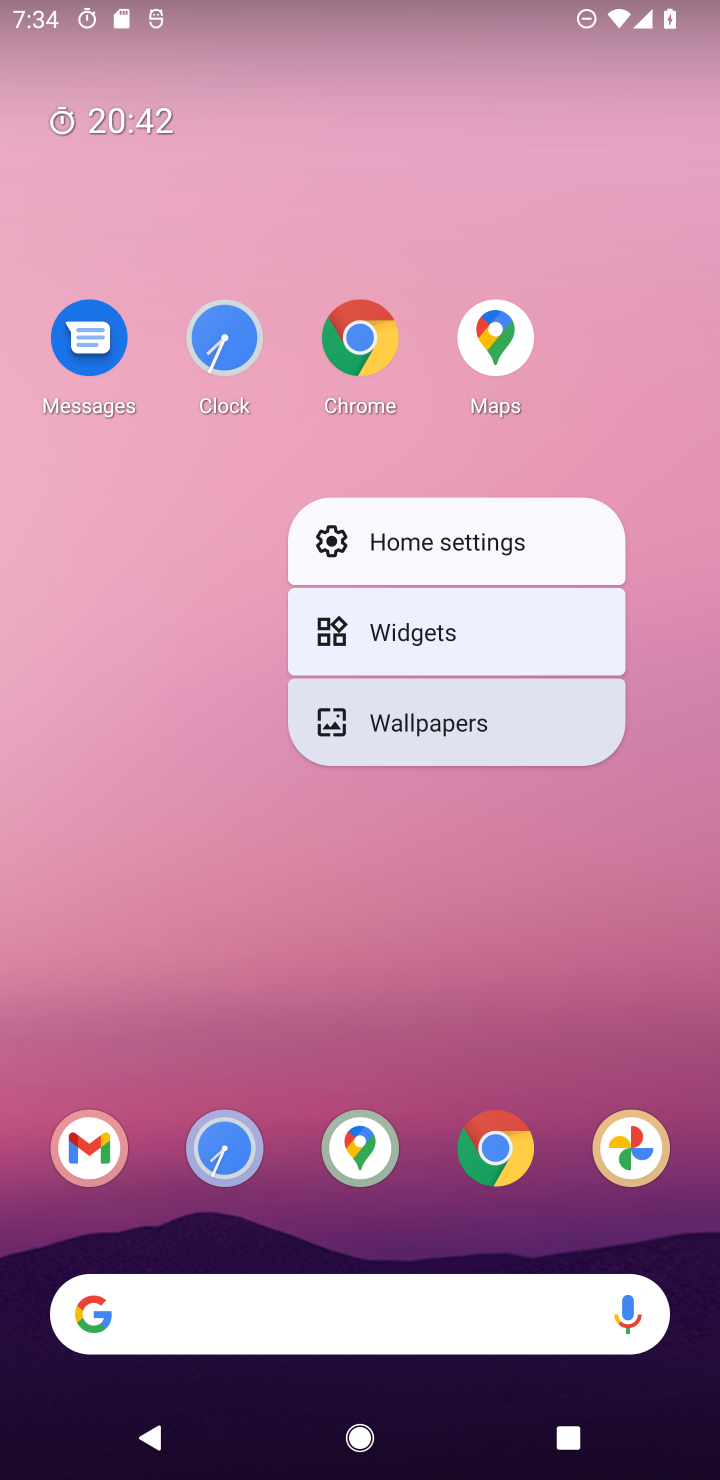
Step 28: drag from (412, 1167) to (425, 305)
Your task to perform on an android device: Open Google Chrome and click the shortcut for Amazon.com Image 29: 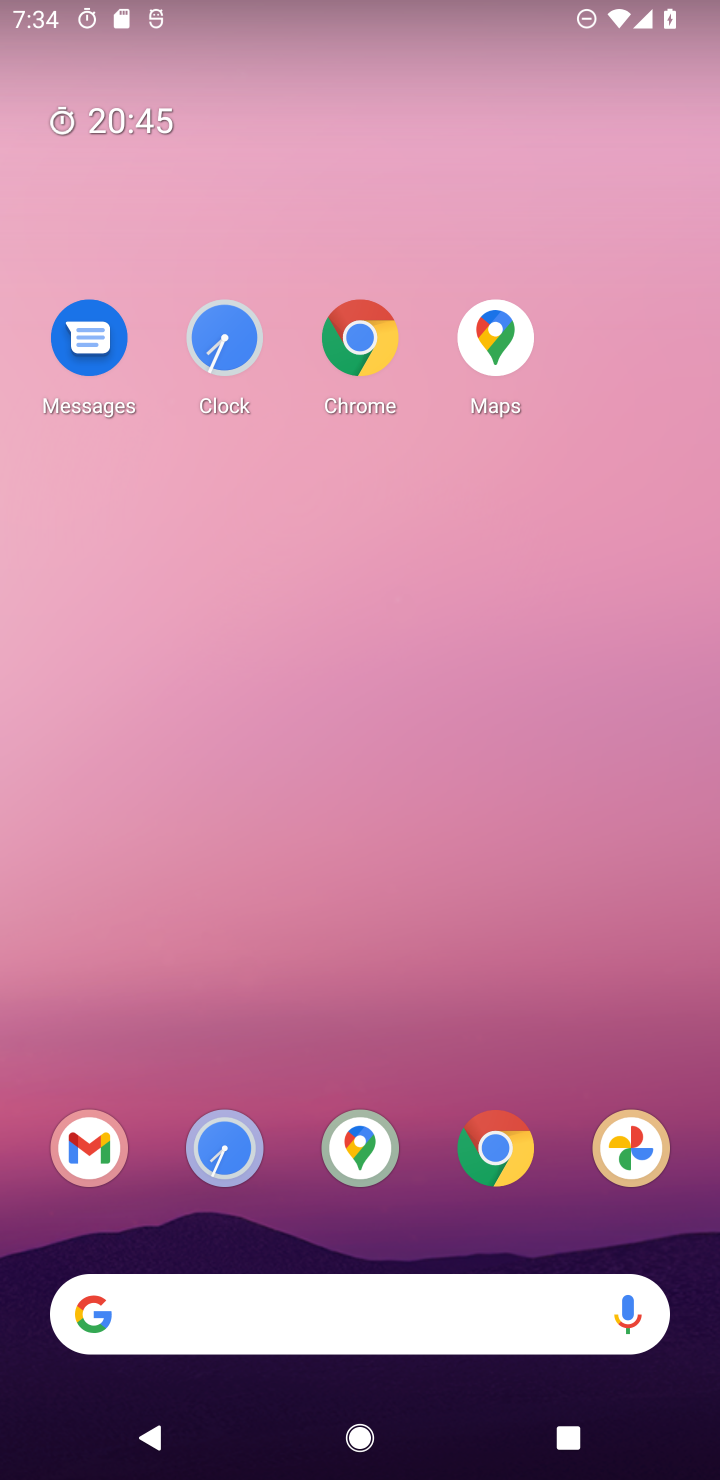
Step 29: drag from (423, 874) to (468, 209)
Your task to perform on an android device: Open Google Chrome and click the shortcut for Amazon.com Image 30: 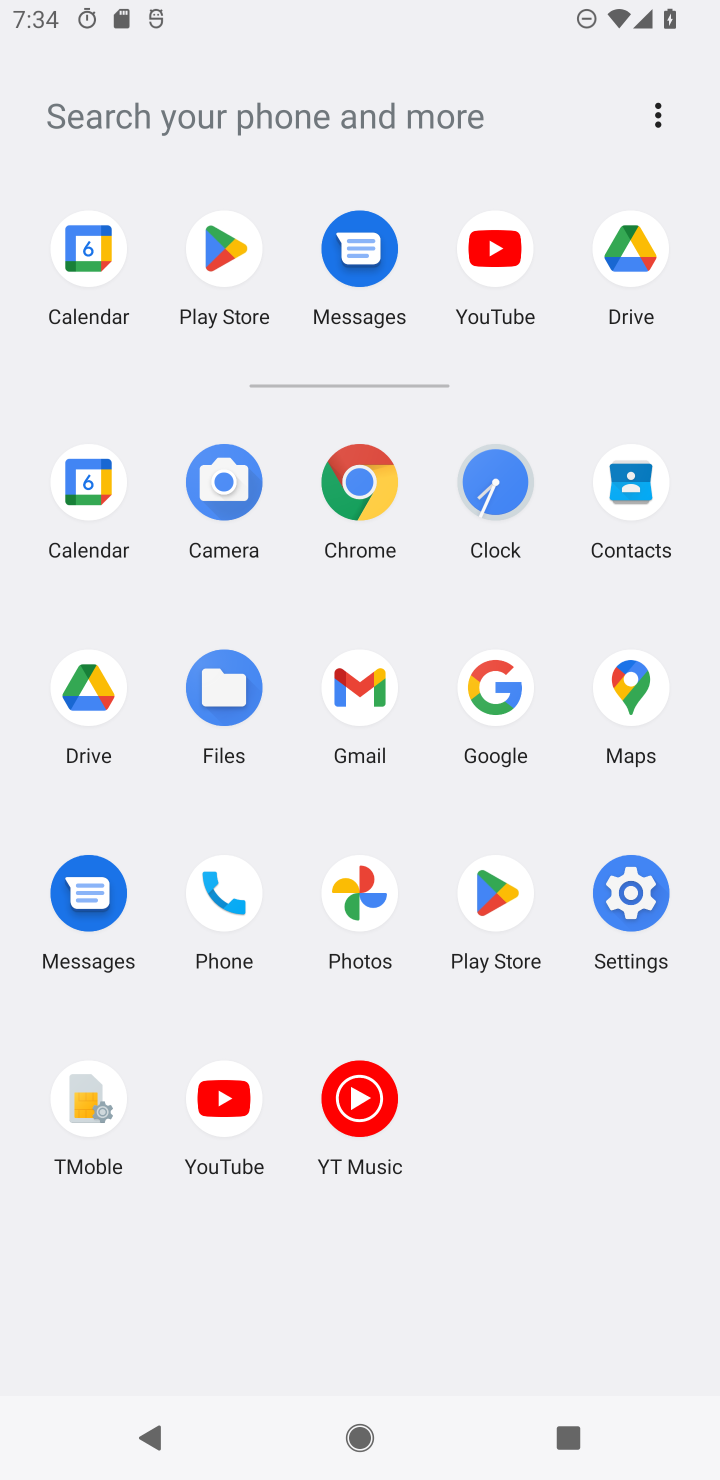
Step 30: click (346, 494)
Your task to perform on an android device: Open Google Chrome and click the shortcut for Amazon.com Image 31: 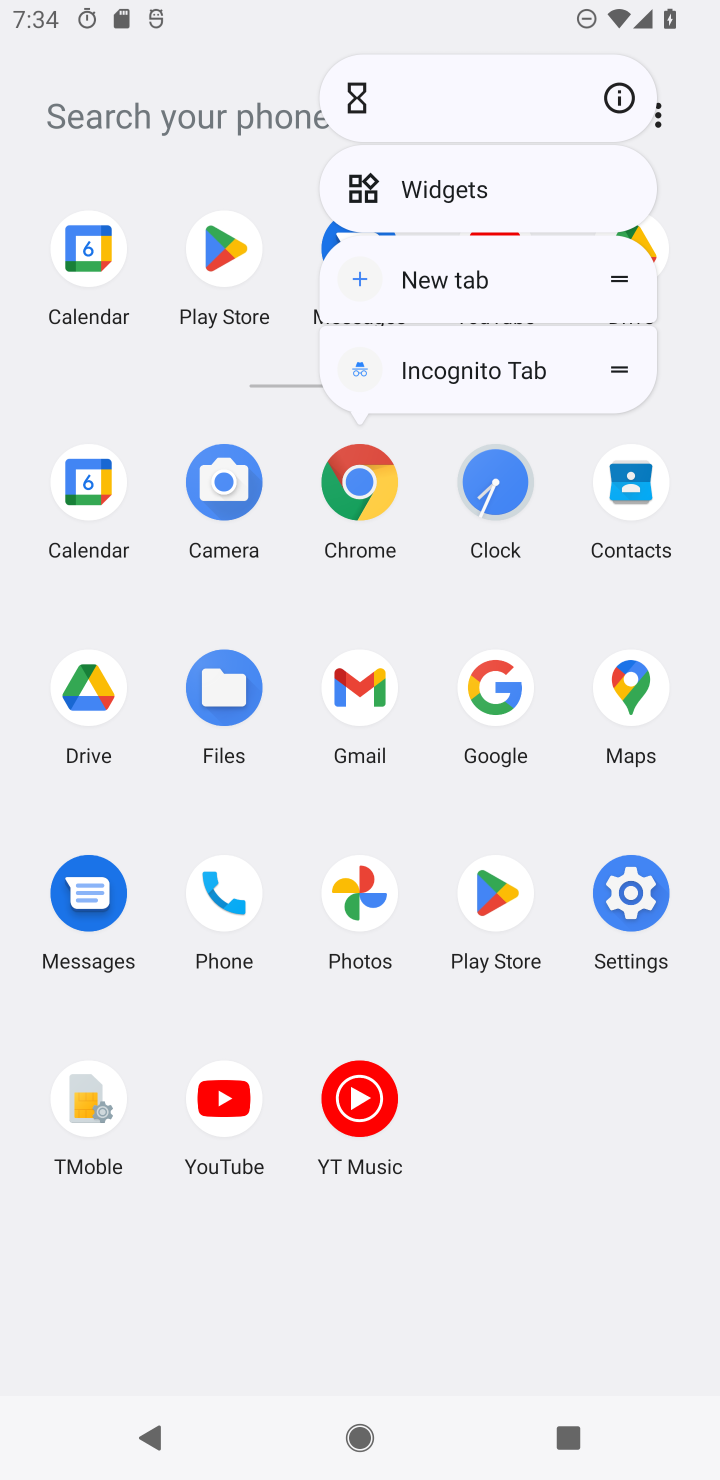
Step 31: click (610, 101)
Your task to perform on an android device: Open Google Chrome and click the shortcut for Amazon.com Image 32: 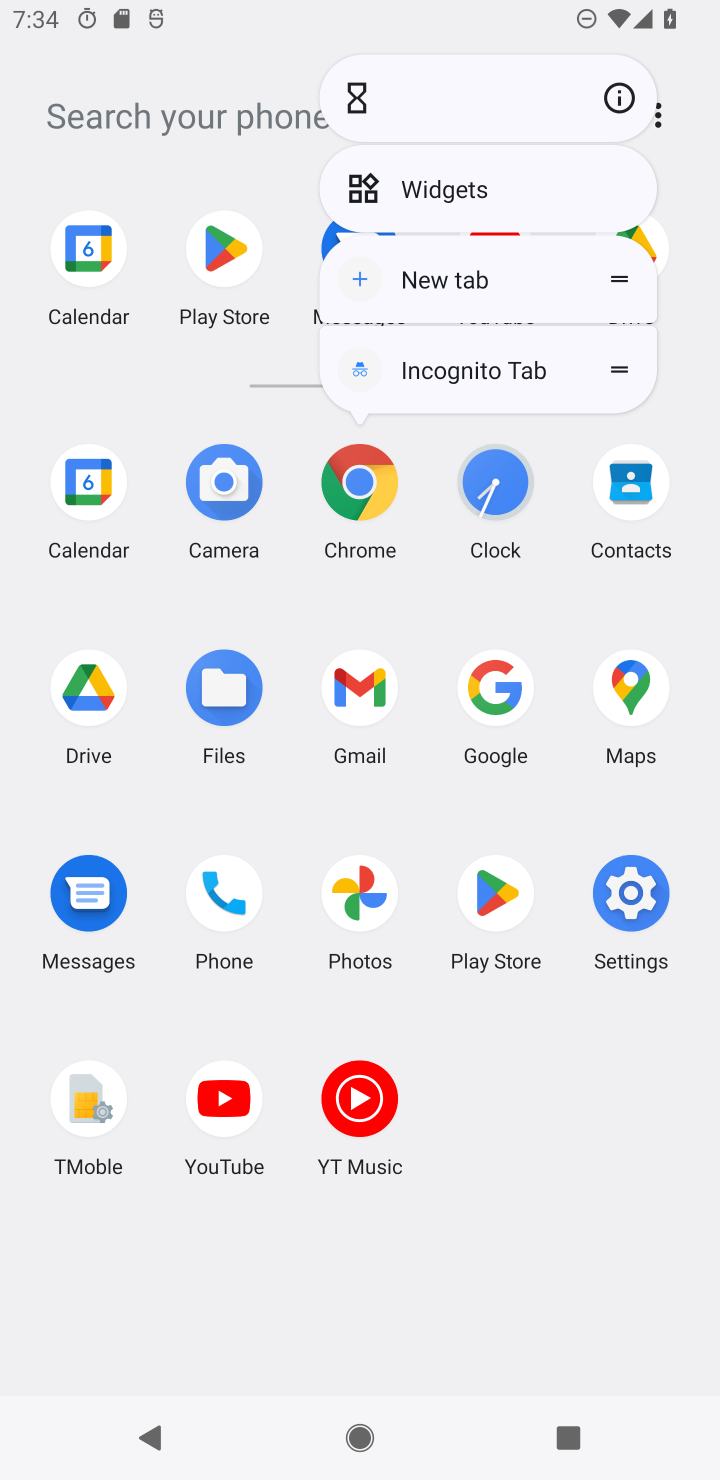
Step 32: click (610, 101)
Your task to perform on an android device: Open Google Chrome and click the shortcut for Amazon.com Image 33: 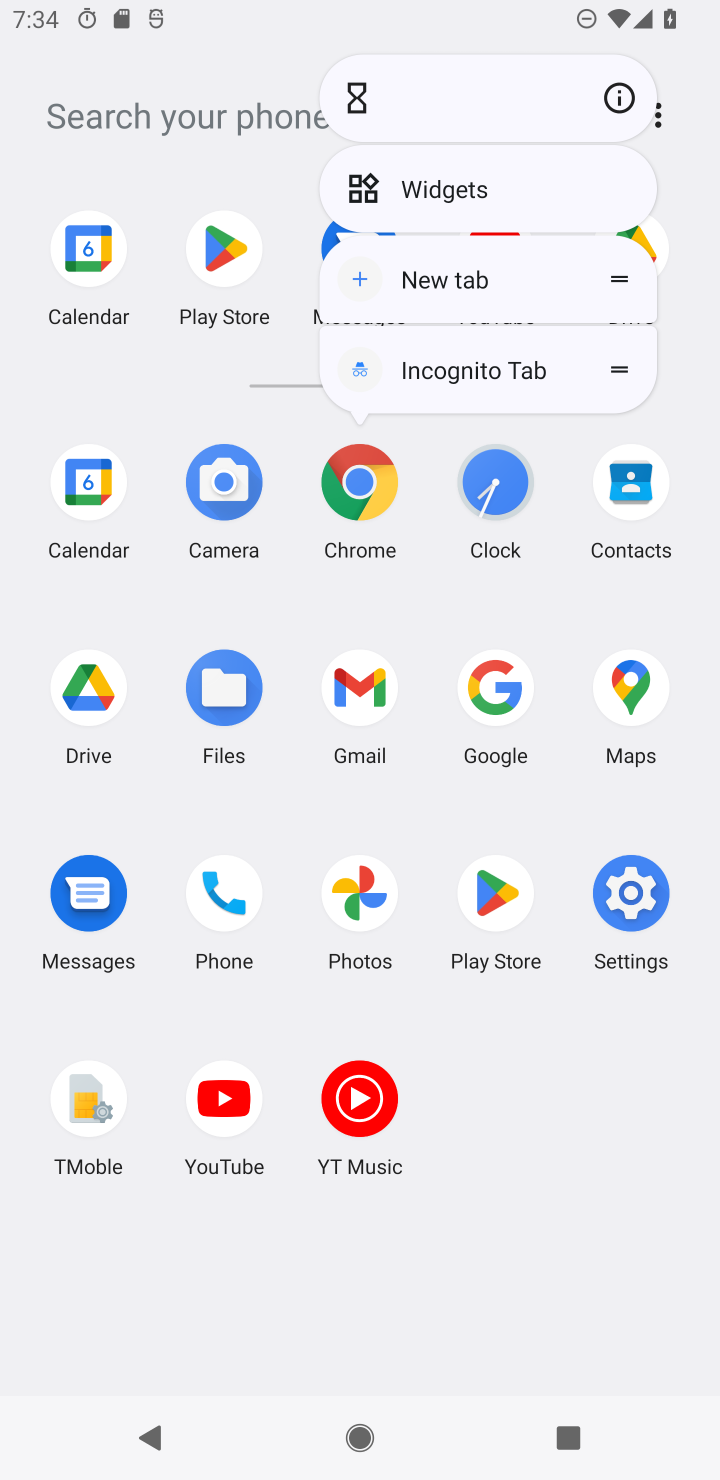
Step 33: click (365, 474)
Your task to perform on an android device: Open Google Chrome and click the shortcut for Amazon.com Image 34: 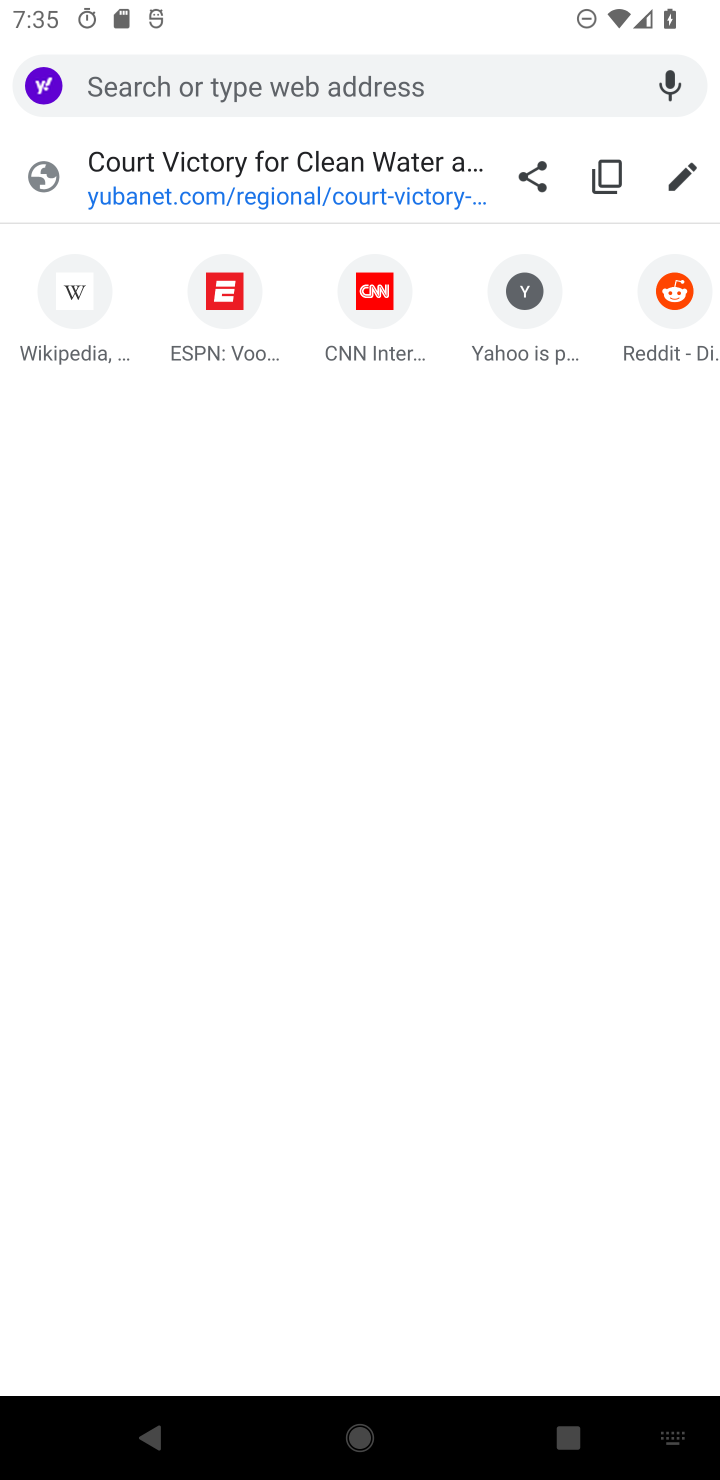
Step 34: drag from (364, 985) to (346, 700)
Your task to perform on an android device: Open Google Chrome and click the shortcut for Amazon.com Image 35: 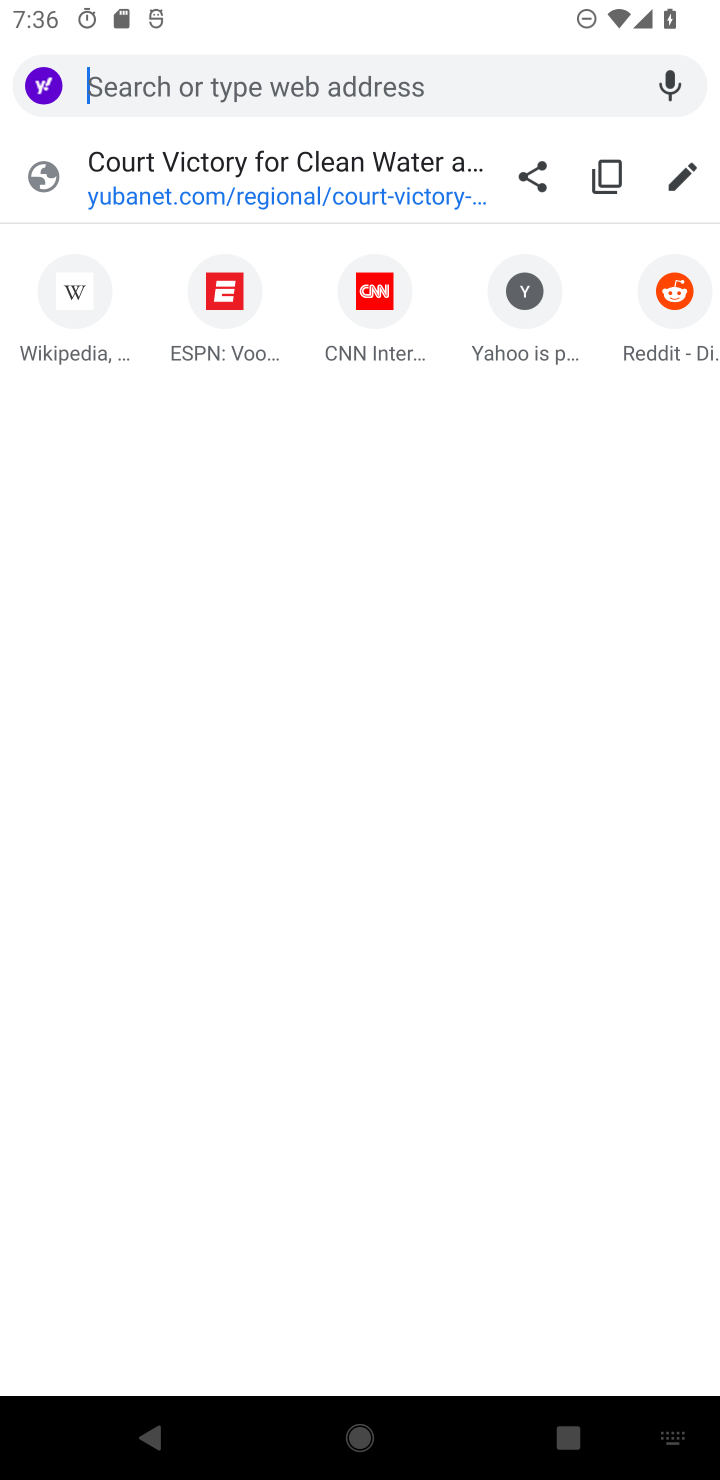
Step 35: drag from (337, 845) to (457, 396)
Your task to perform on an android device: Open Google Chrome and click the shortcut for Amazon.com Image 36: 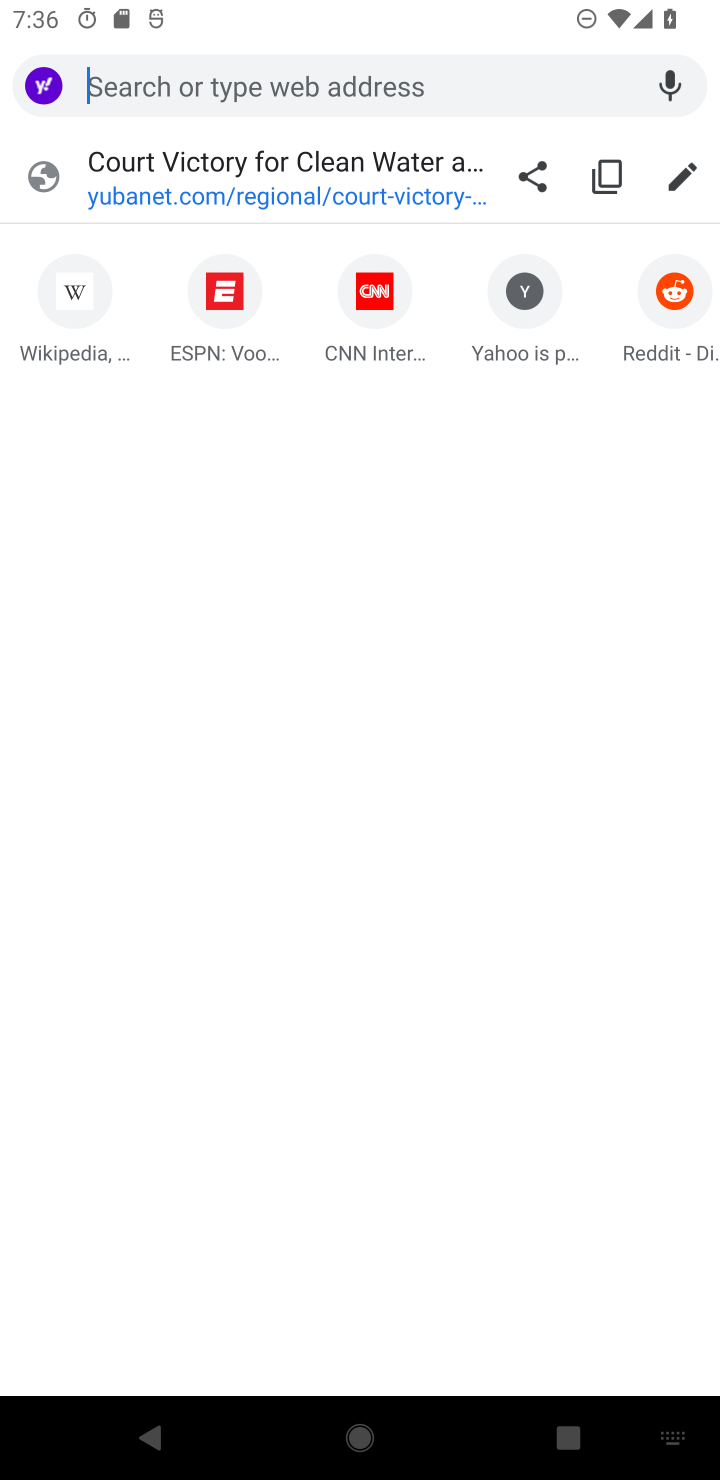
Step 36: press home button
Your task to perform on an android device: Open Google Chrome and click the shortcut for Amazon.com Image 37: 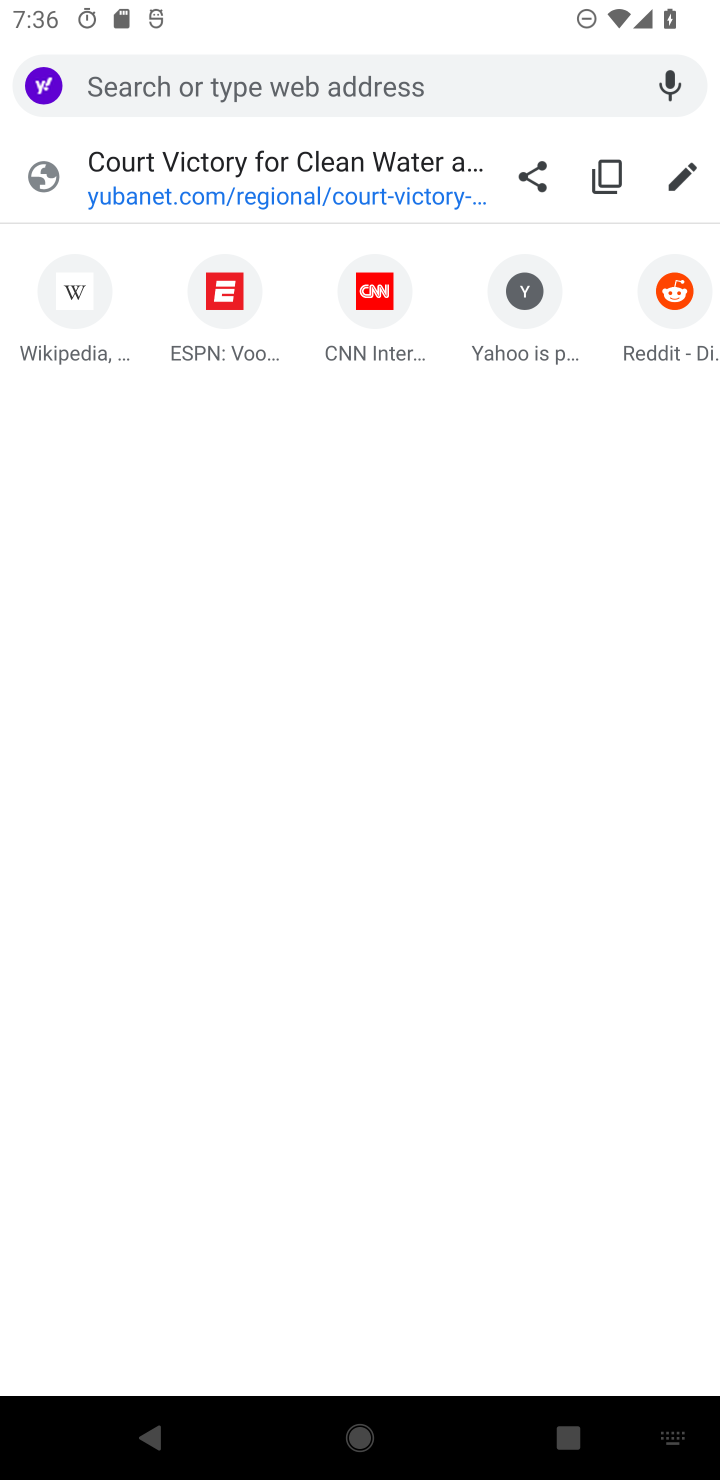
Step 37: click (524, 212)
Your task to perform on an android device: Open Google Chrome and click the shortcut for Amazon.com Image 38: 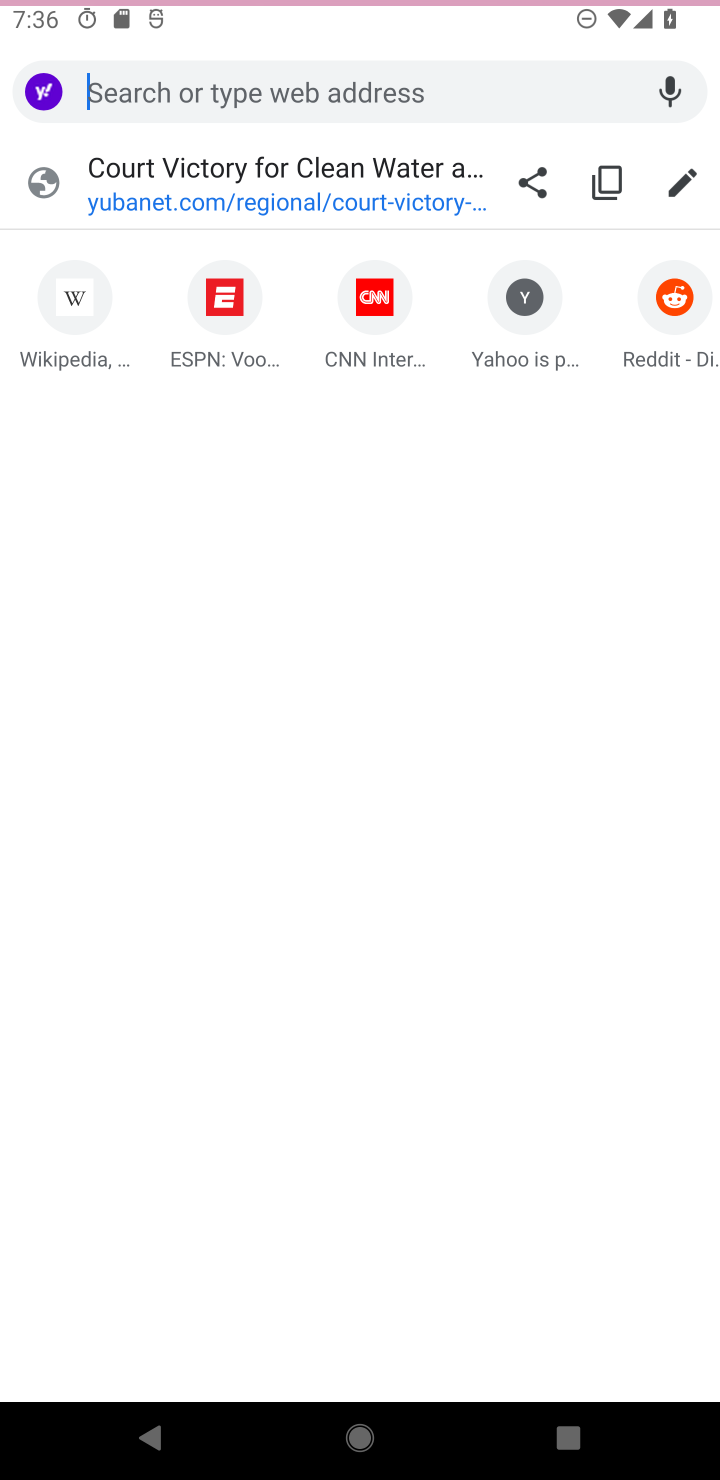
Step 38: drag from (338, 738) to (487, 240)
Your task to perform on an android device: Open Google Chrome and click the shortcut for Amazon.com Image 39: 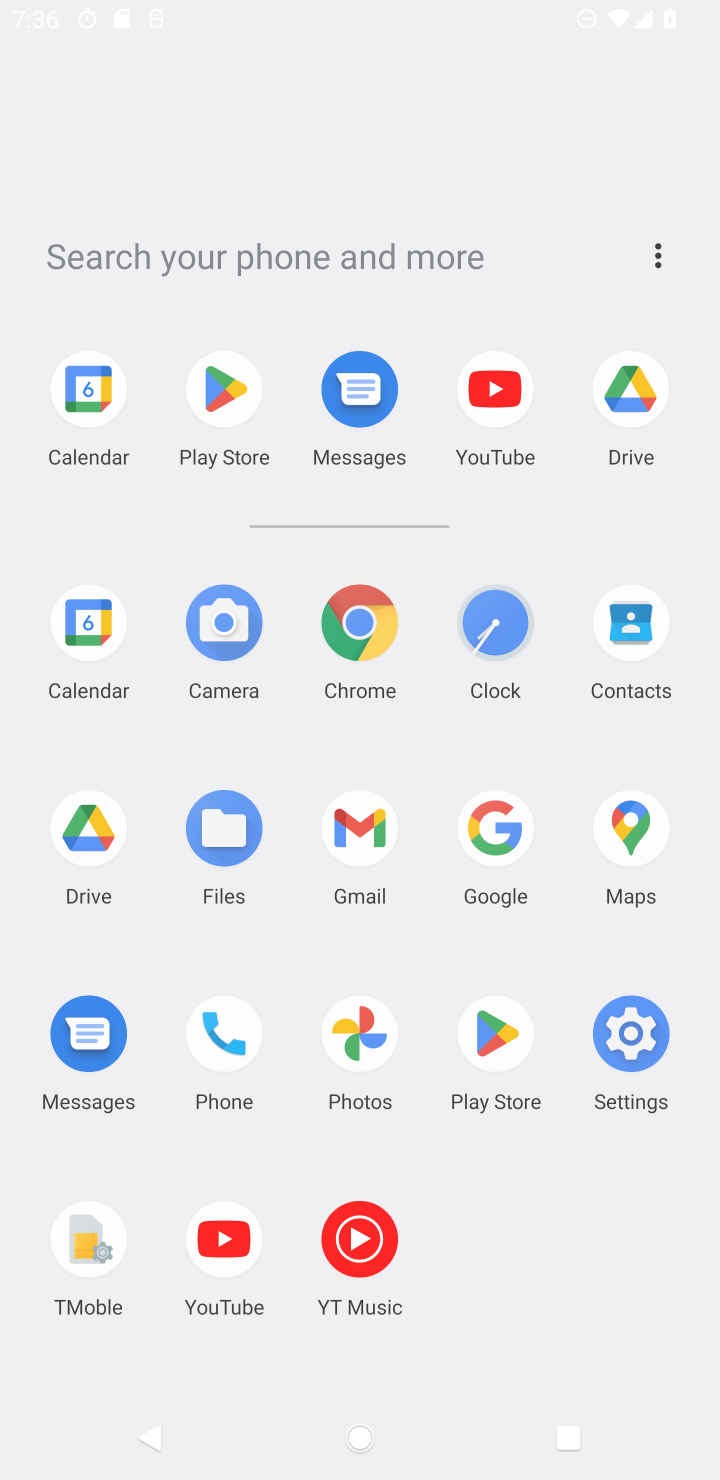
Step 39: press home button
Your task to perform on an android device: Open Google Chrome and click the shortcut for Amazon.com Image 40: 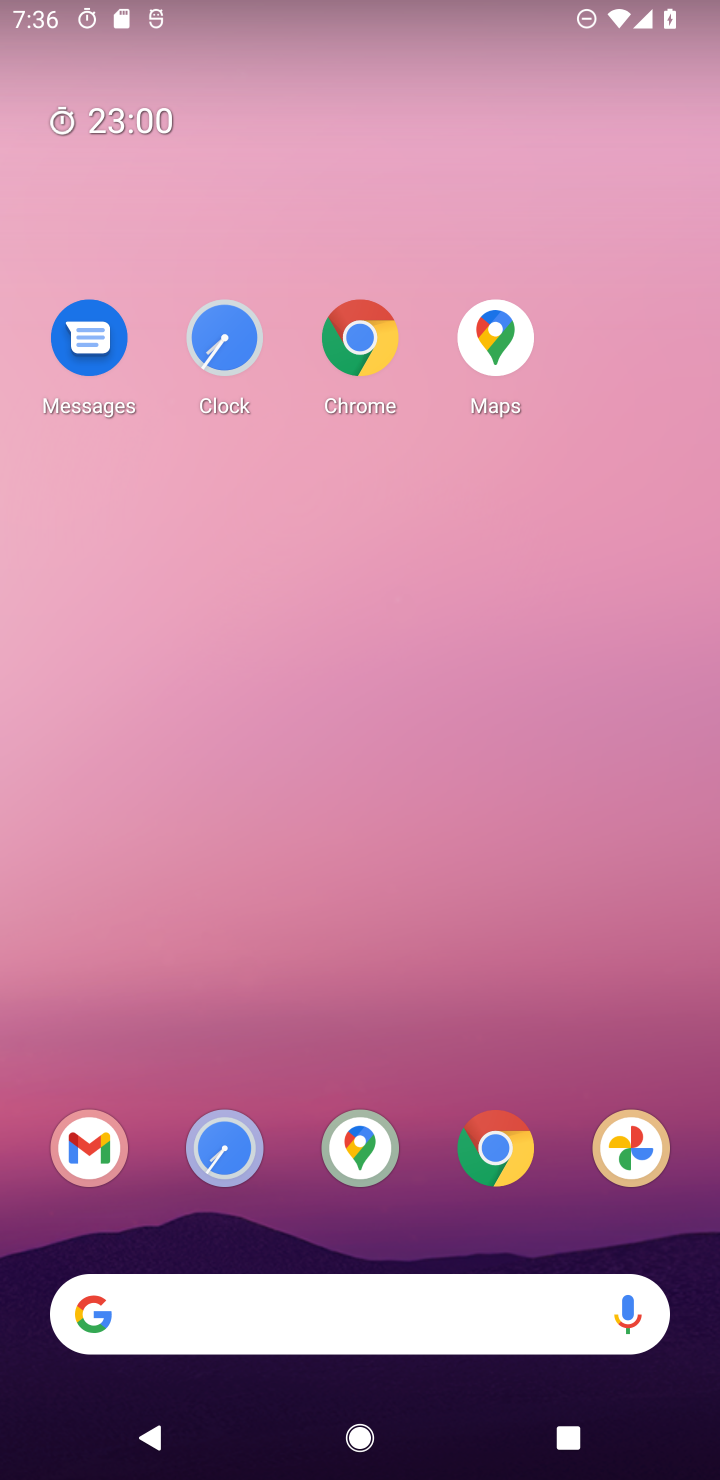
Step 40: click (355, 337)
Your task to perform on an android device: Open Google Chrome and click the shortcut for Amazon.com Image 41: 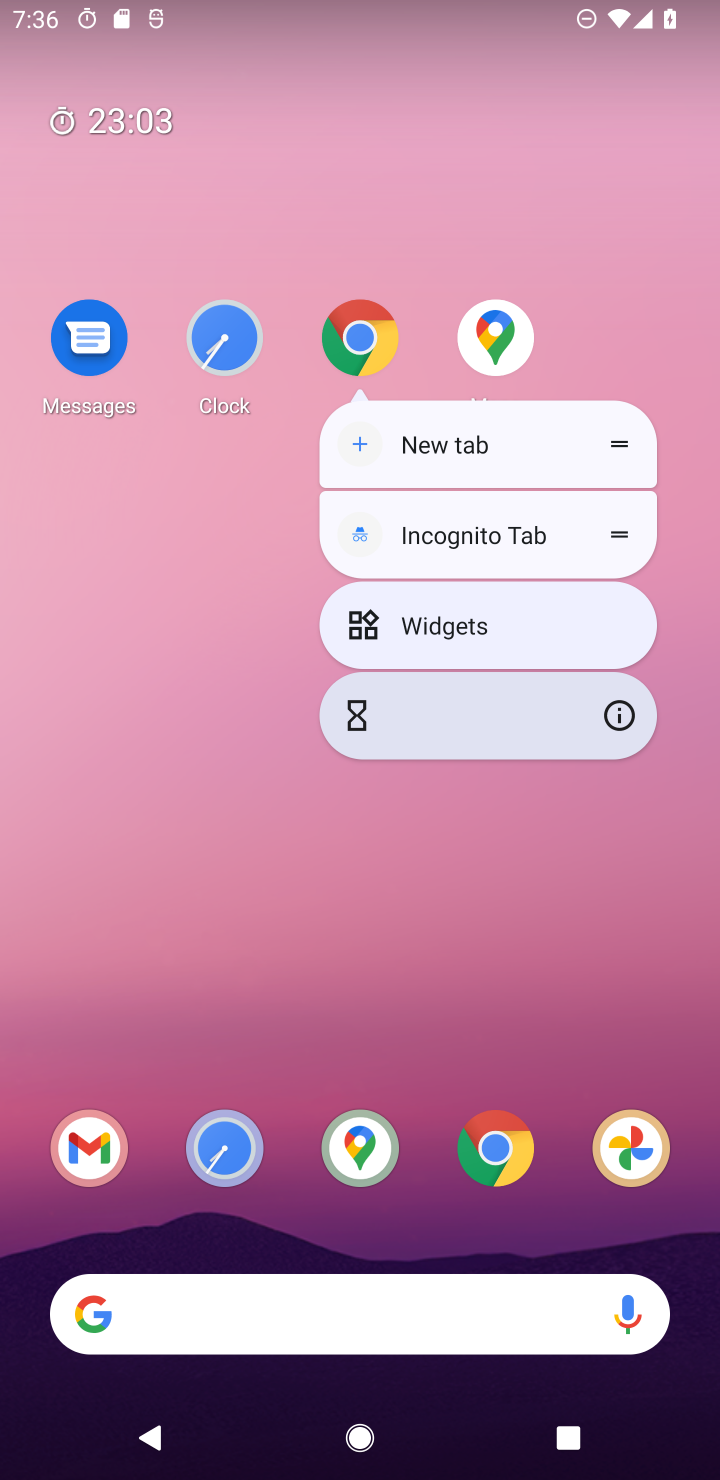
Step 41: click (604, 720)
Your task to perform on an android device: Open Google Chrome and click the shortcut for Amazon.com Image 42: 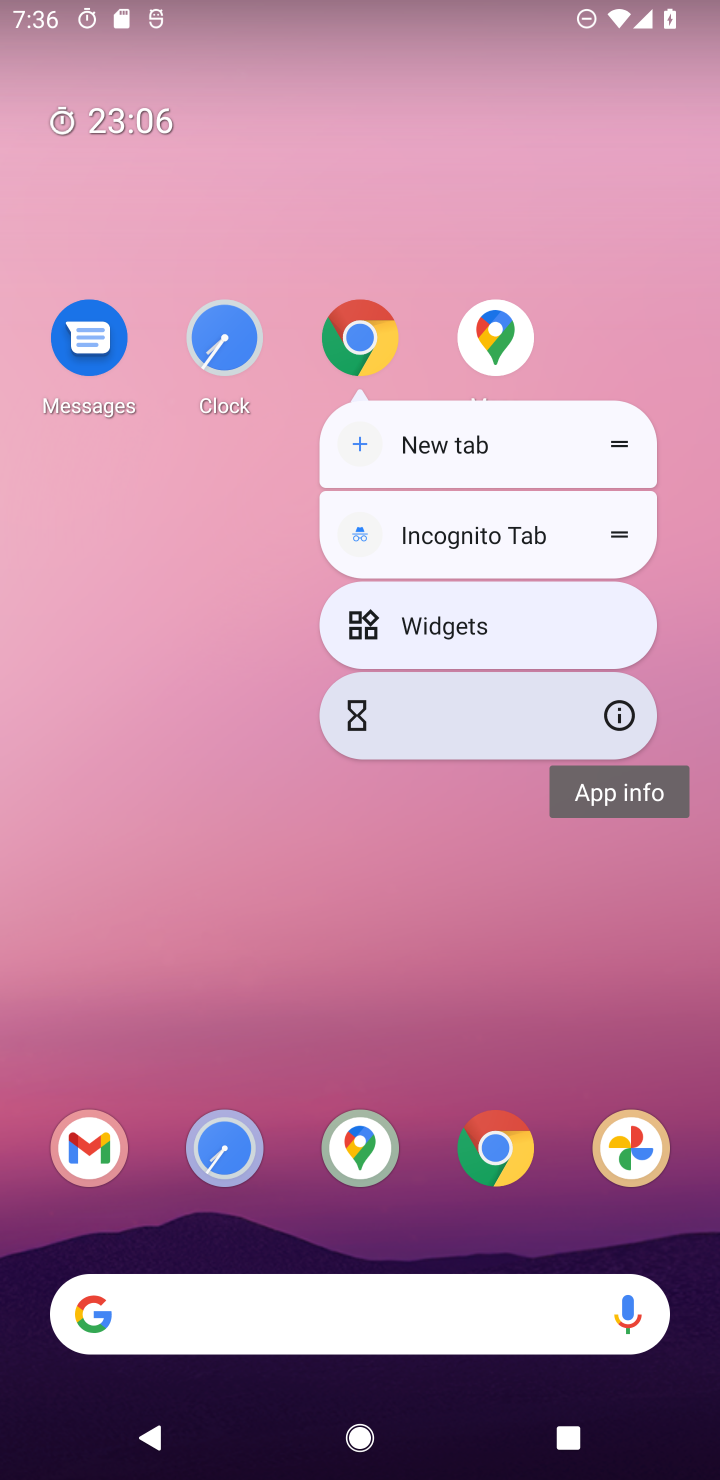
Step 42: click (604, 720)
Your task to perform on an android device: Open Google Chrome and click the shortcut for Amazon.com Image 43: 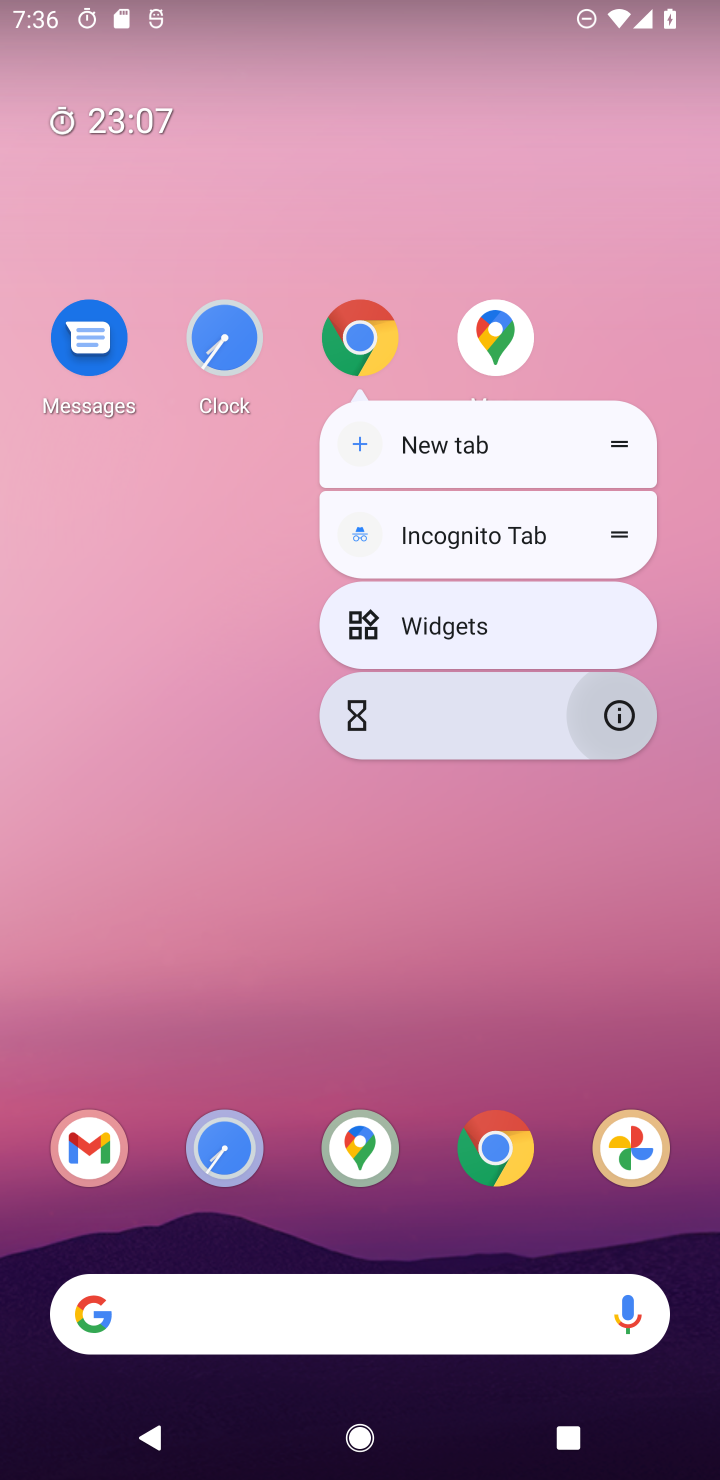
Step 43: click (349, 341)
Your task to perform on an android device: Open Google Chrome and click the shortcut for Amazon.com Image 44: 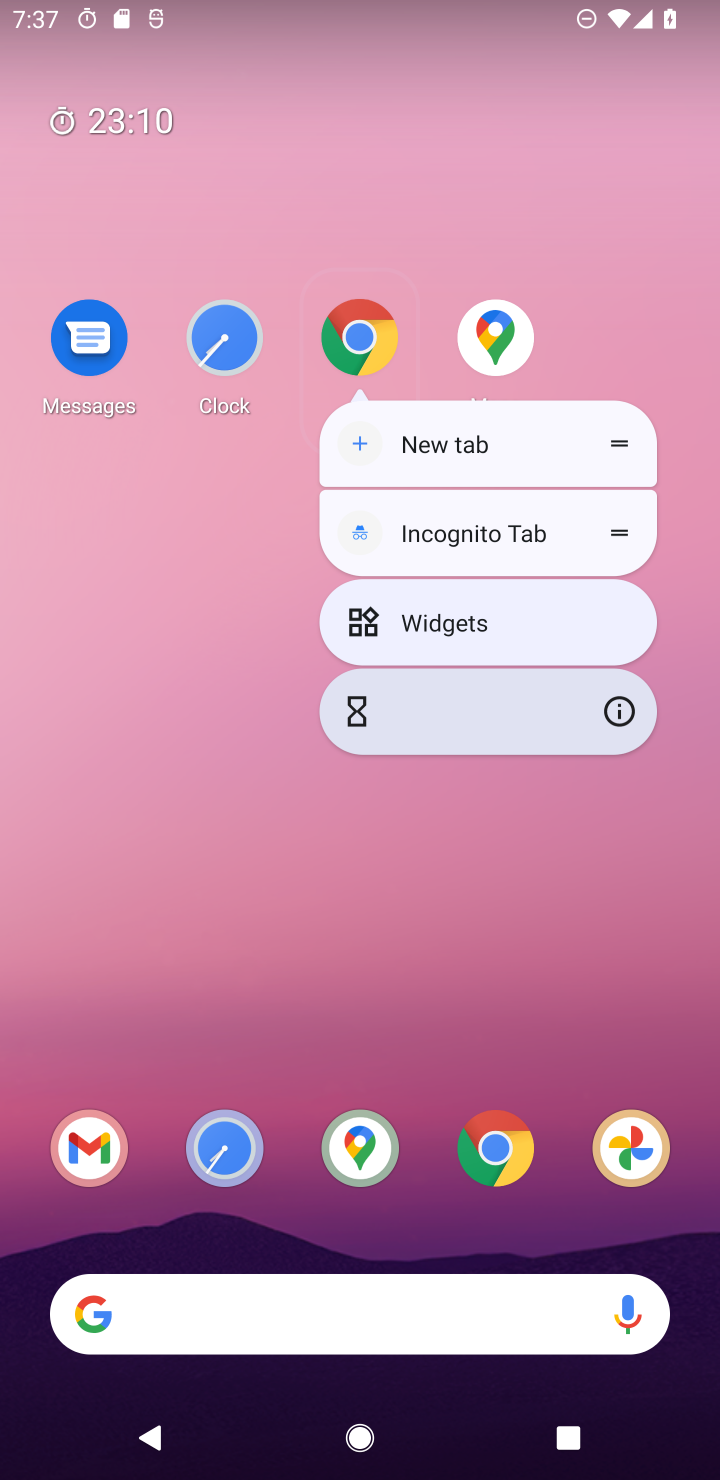
Step 44: click (349, 341)
Your task to perform on an android device: Open Google Chrome and click the shortcut for Amazon.com Image 45: 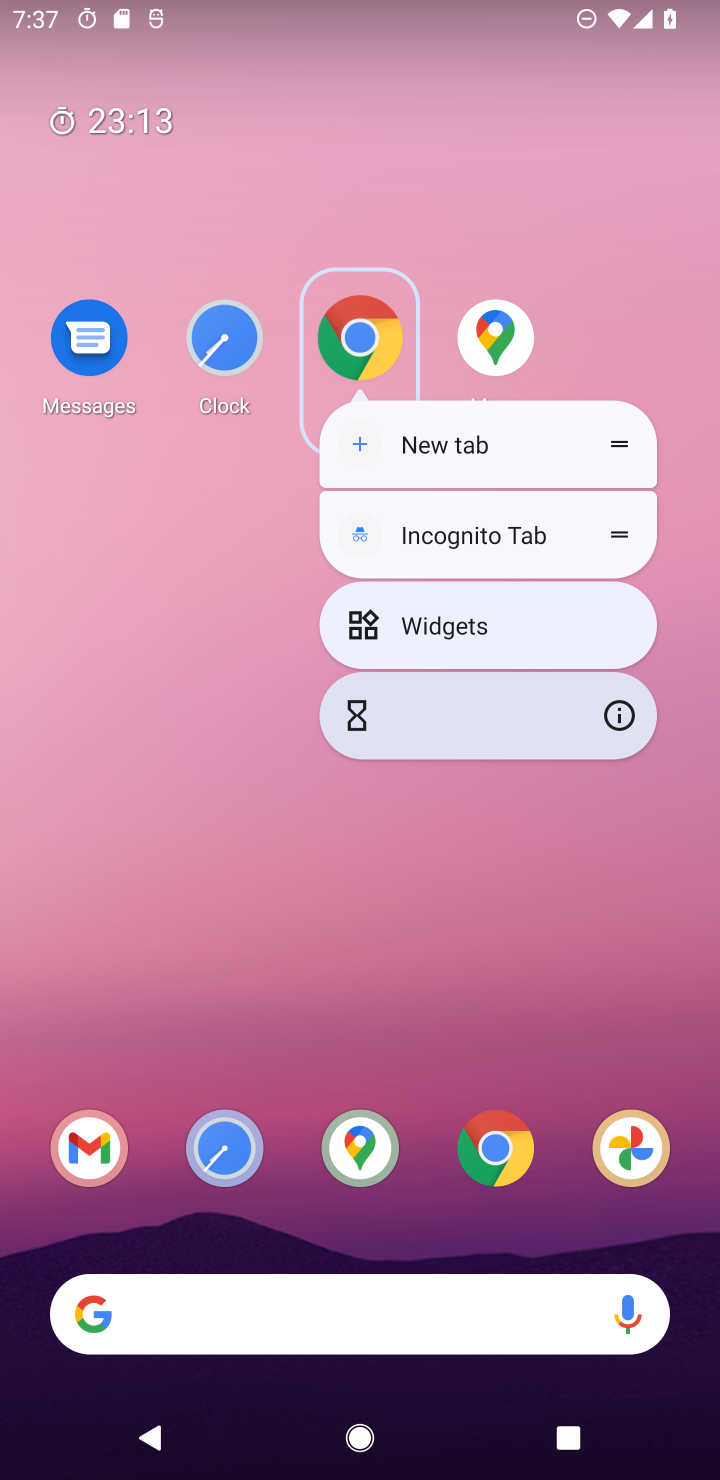
Step 45: click (349, 341)
Your task to perform on an android device: Open Google Chrome and click the shortcut for Amazon.com Image 46: 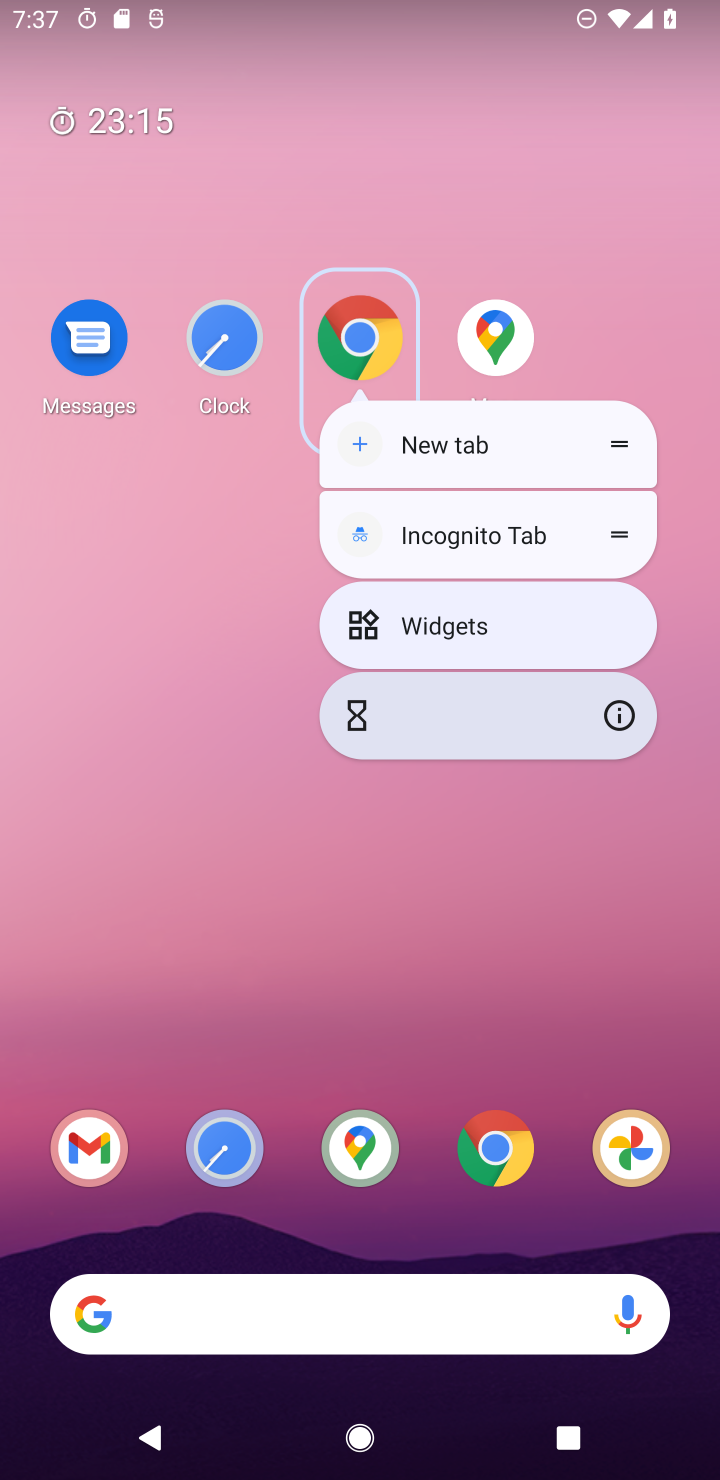
Step 46: click (349, 341)
Your task to perform on an android device: Open Google Chrome and click the shortcut for Amazon.com Image 47: 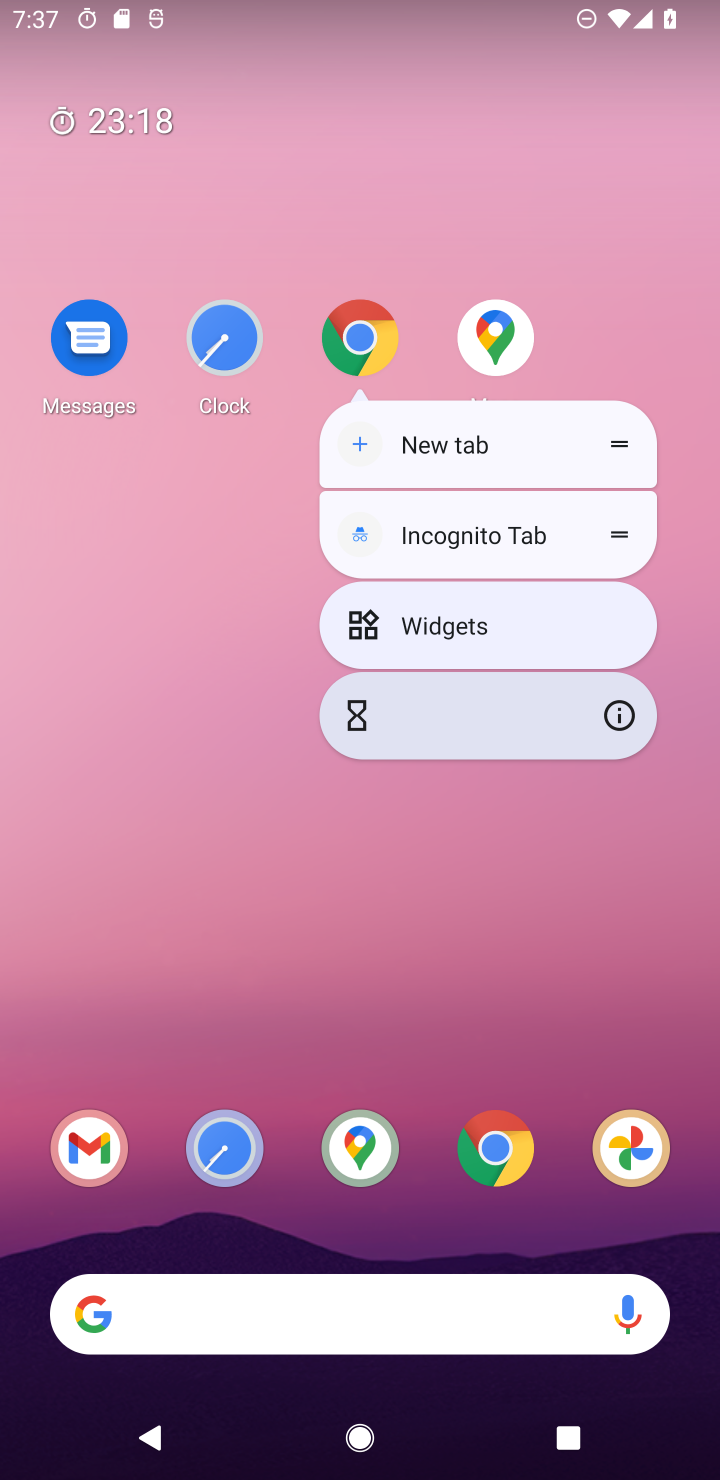
Step 47: click (618, 700)
Your task to perform on an android device: Open Google Chrome and click the shortcut for Amazon.com Image 48: 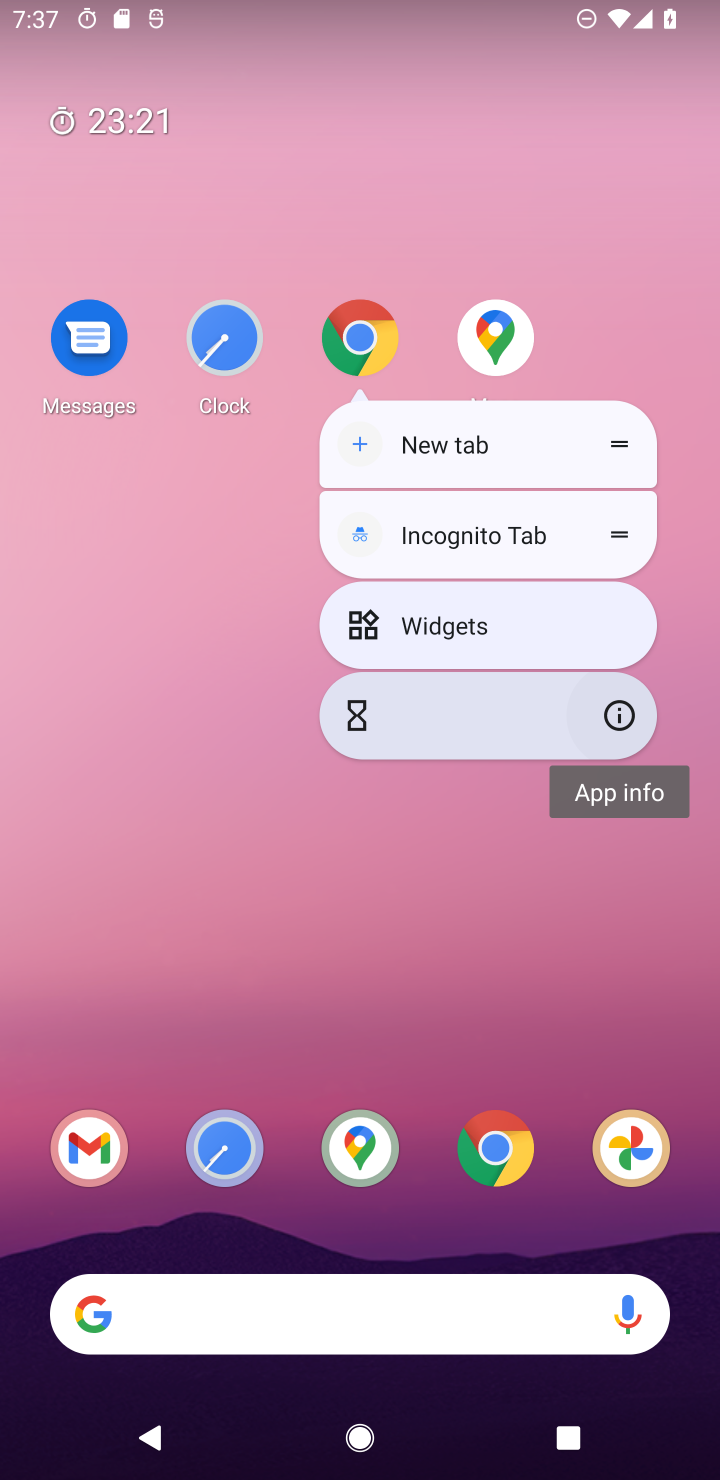
Step 48: click (618, 700)
Your task to perform on an android device: Open Google Chrome and click the shortcut for Amazon.com Image 49: 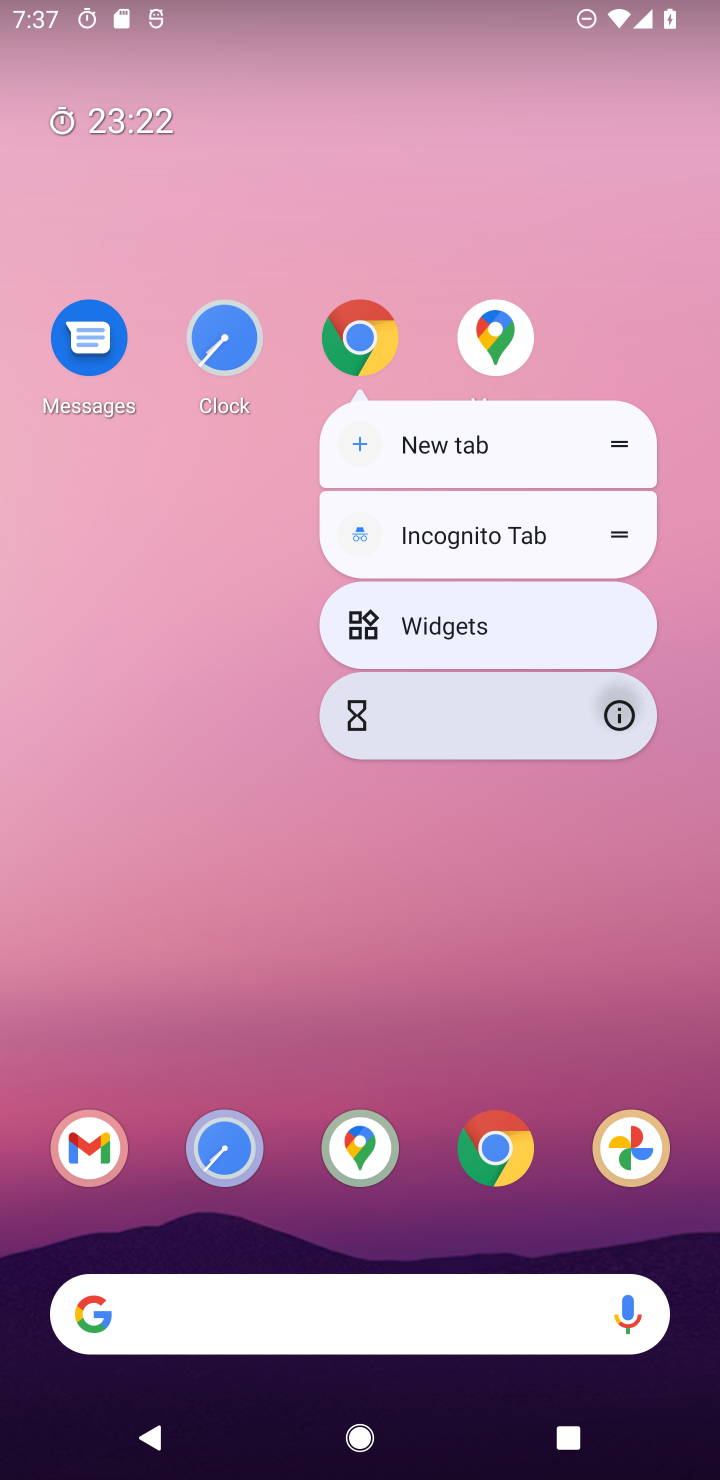
Step 49: click (614, 702)
Your task to perform on an android device: Open Google Chrome and click the shortcut for Amazon.com Image 50: 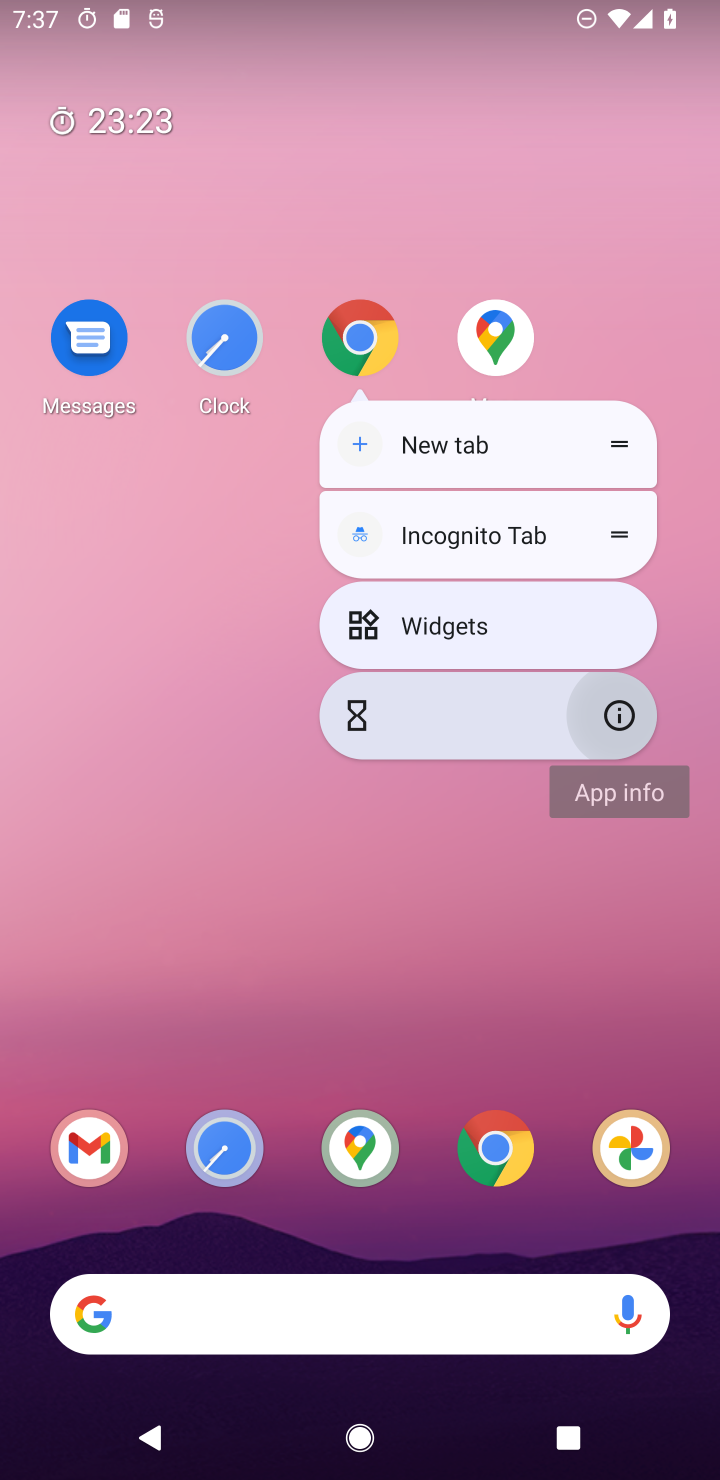
Step 50: click (614, 702)
Your task to perform on an android device: Open Google Chrome and click the shortcut for Amazon.com Image 51: 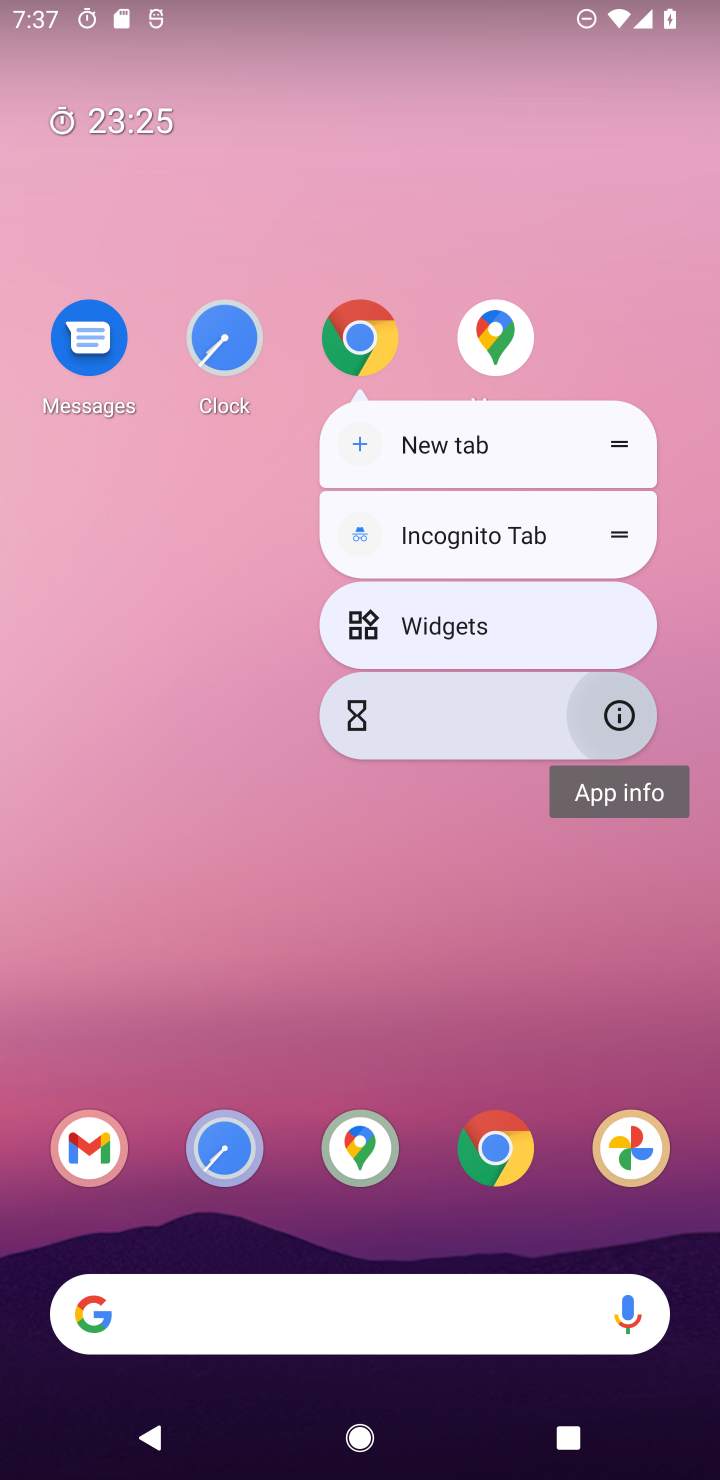
Step 51: click (618, 709)
Your task to perform on an android device: Open Google Chrome and click the shortcut for Amazon.com Image 52: 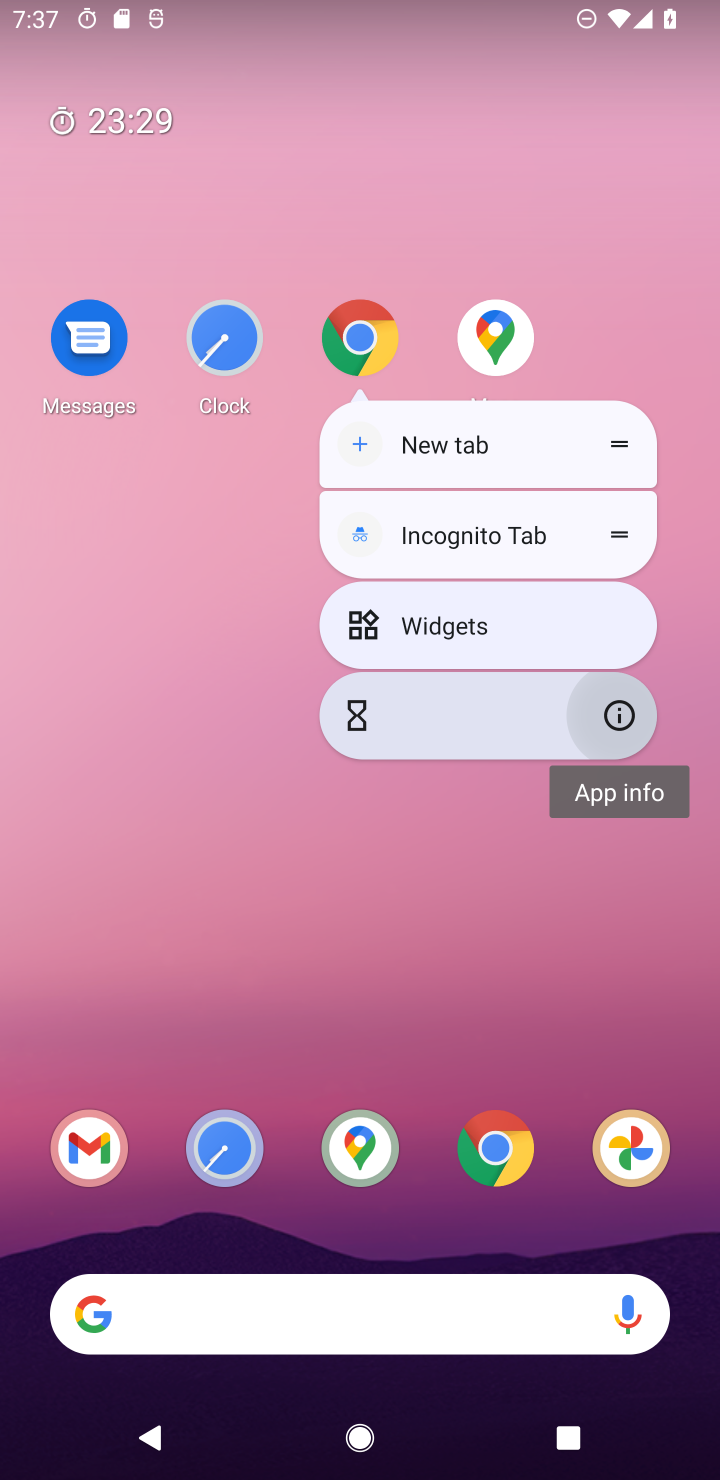
Step 52: click (342, 333)
Your task to perform on an android device: Open Google Chrome and click the shortcut for Amazon.com Image 53: 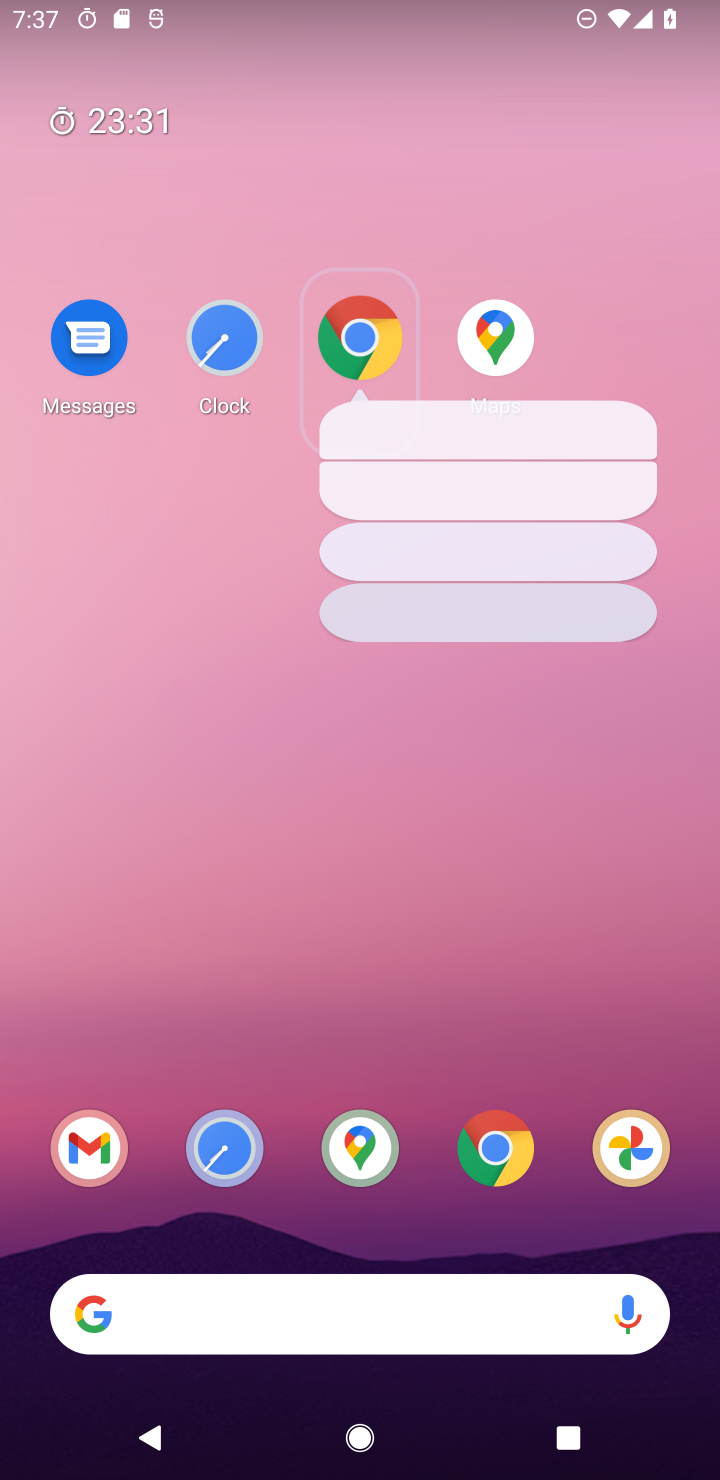
Step 53: click (342, 333)
Your task to perform on an android device: Open Google Chrome and click the shortcut for Amazon.com Image 54: 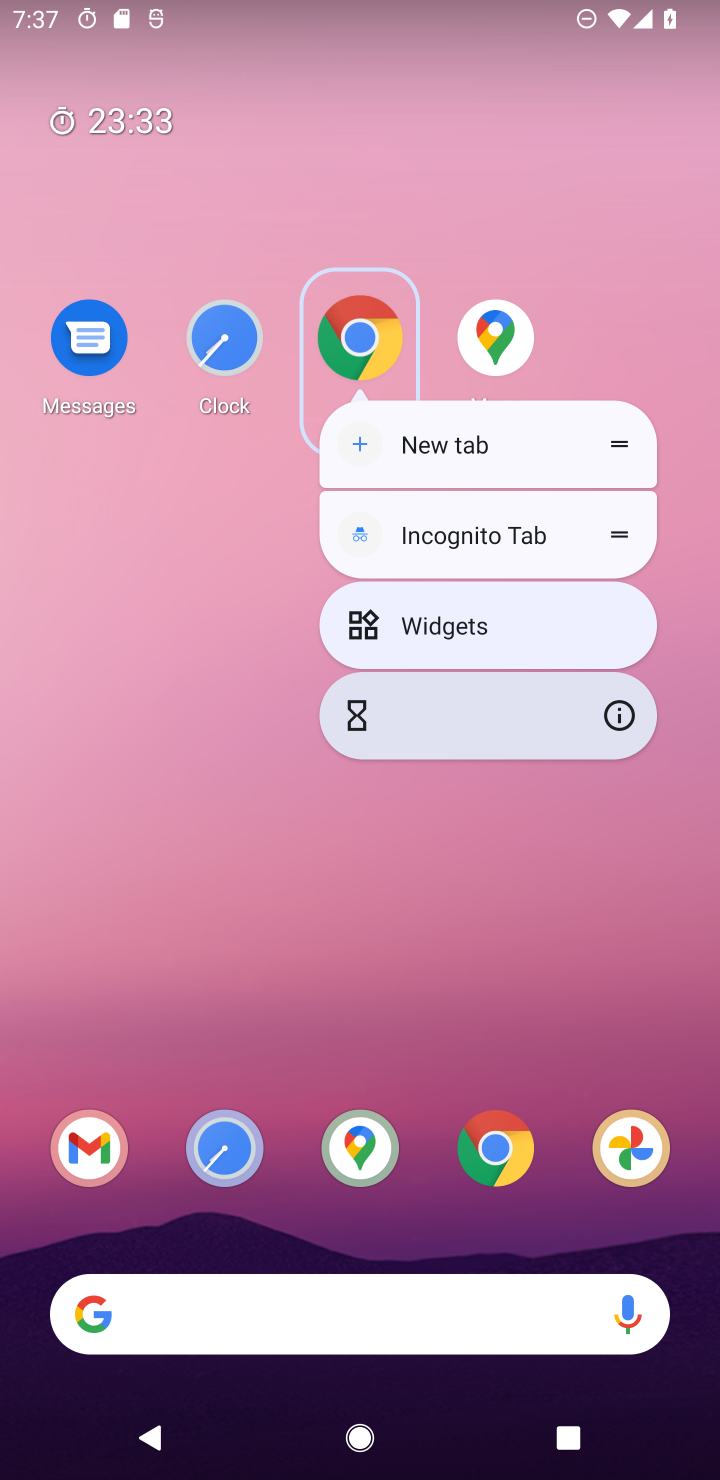
Step 54: click (504, 1141)
Your task to perform on an android device: Open Google Chrome and click the shortcut for Amazon.com Image 55: 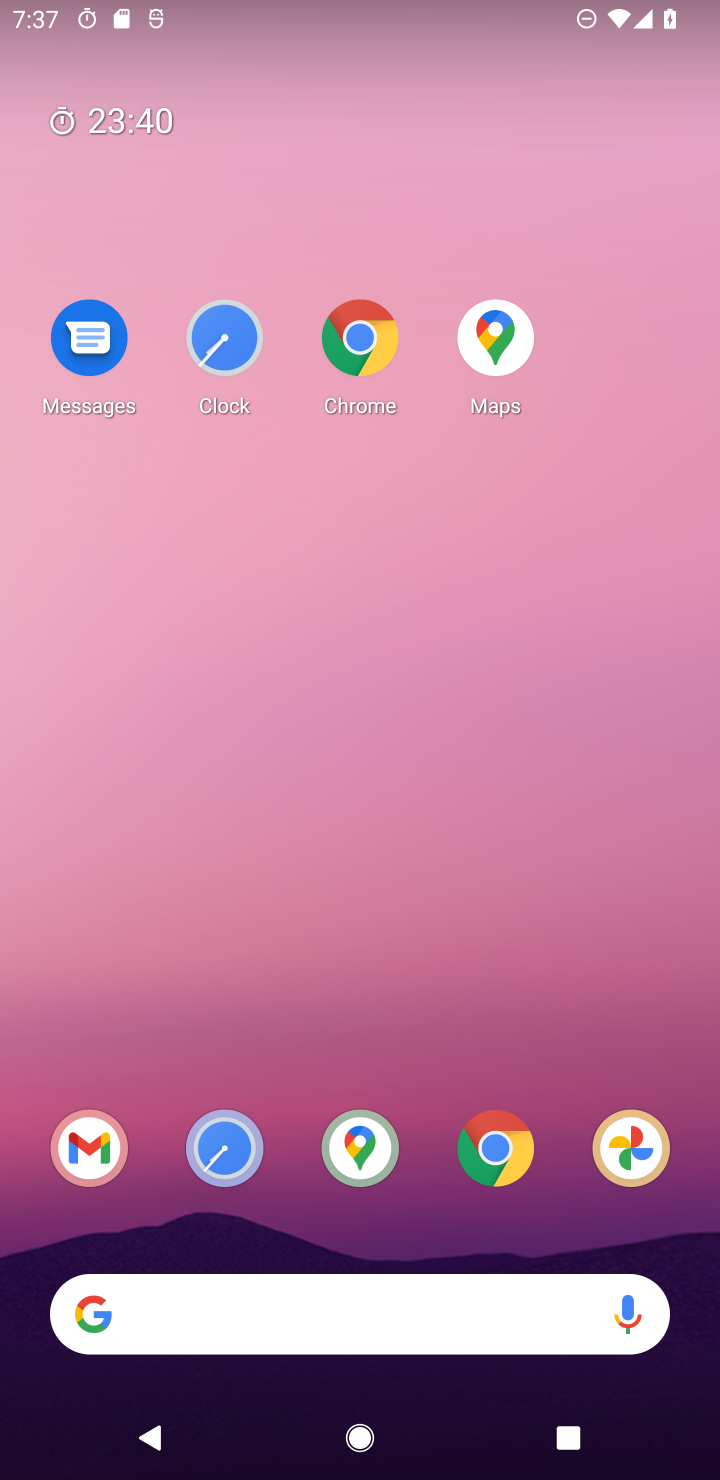
Step 55: drag from (526, 266) to (577, 35)
Your task to perform on an android device: Open Google Chrome and click the shortcut for Amazon.com Image 56: 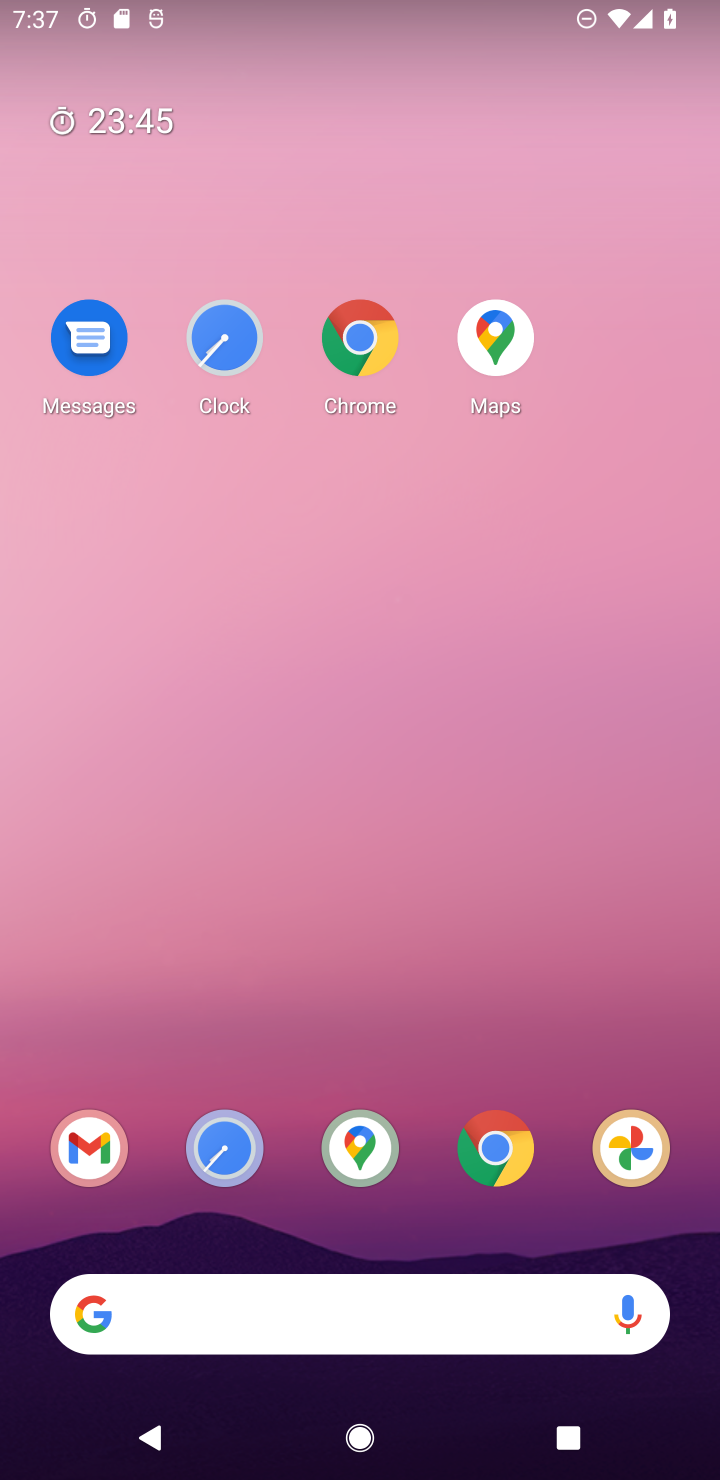
Step 56: click (488, 1147)
Your task to perform on an android device: Open Google Chrome and click the shortcut for Amazon.com Image 57: 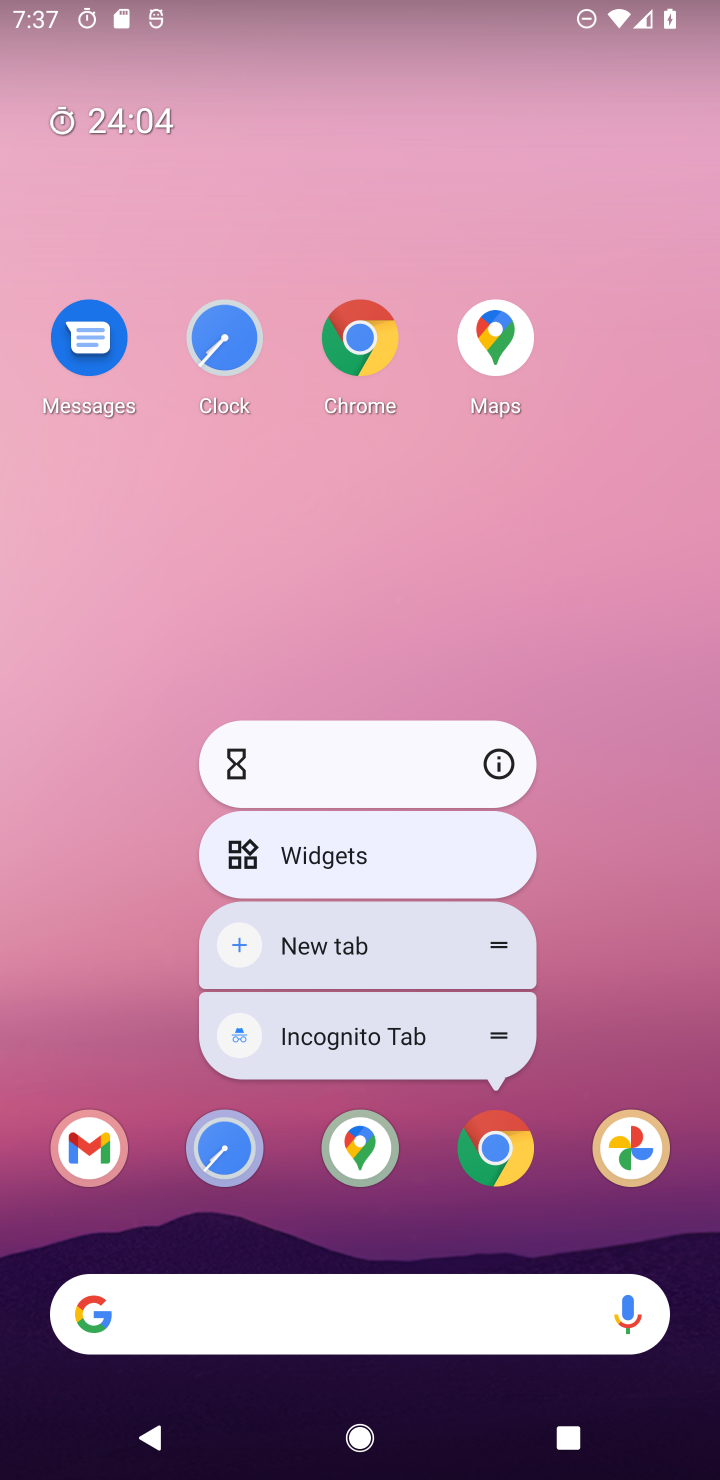
Step 57: click (490, 1135)
Your task to perform on an android device: Open Google Chrome and click the shortcut for Amazon.com Image 58: 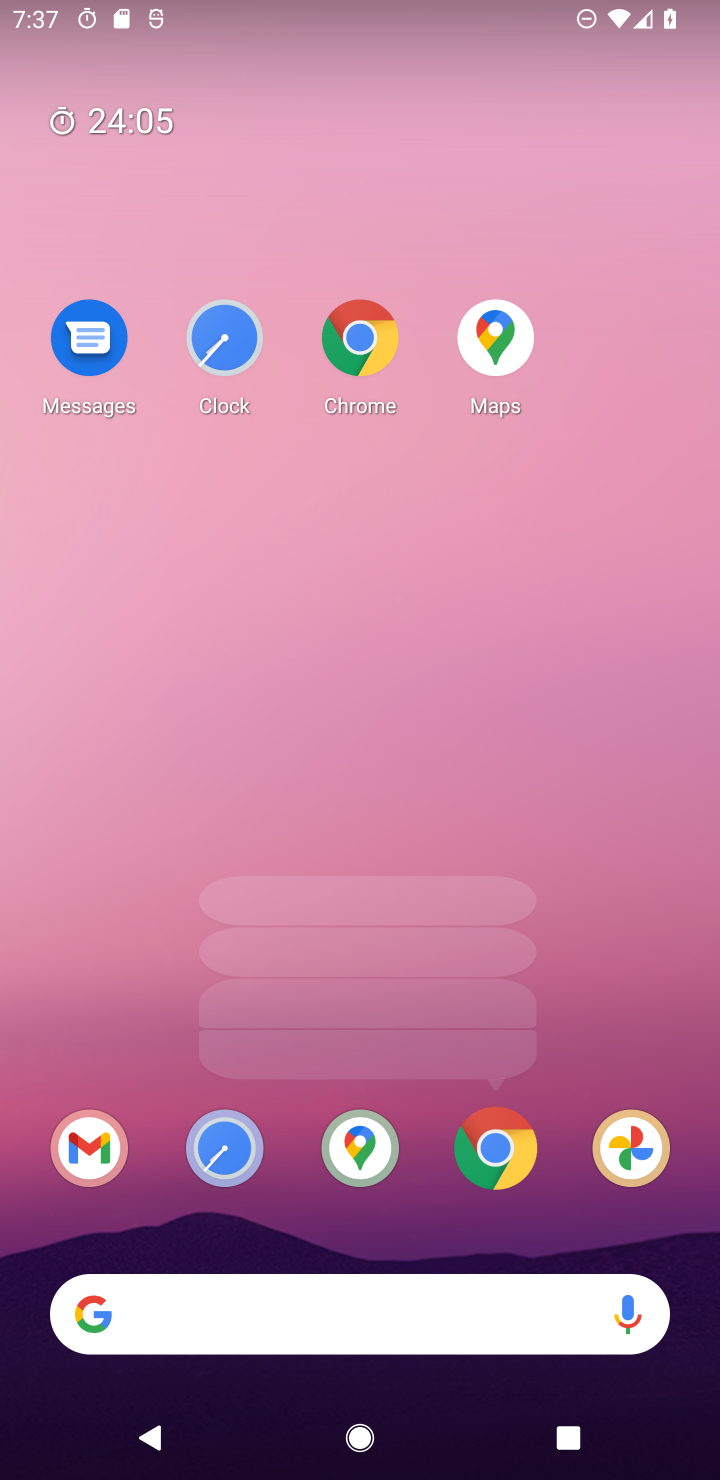
Step 58: click (505, 738)
Your task to perform on an android device: Open Google Chrome and click the shortcut for Amazon.com Image 59: 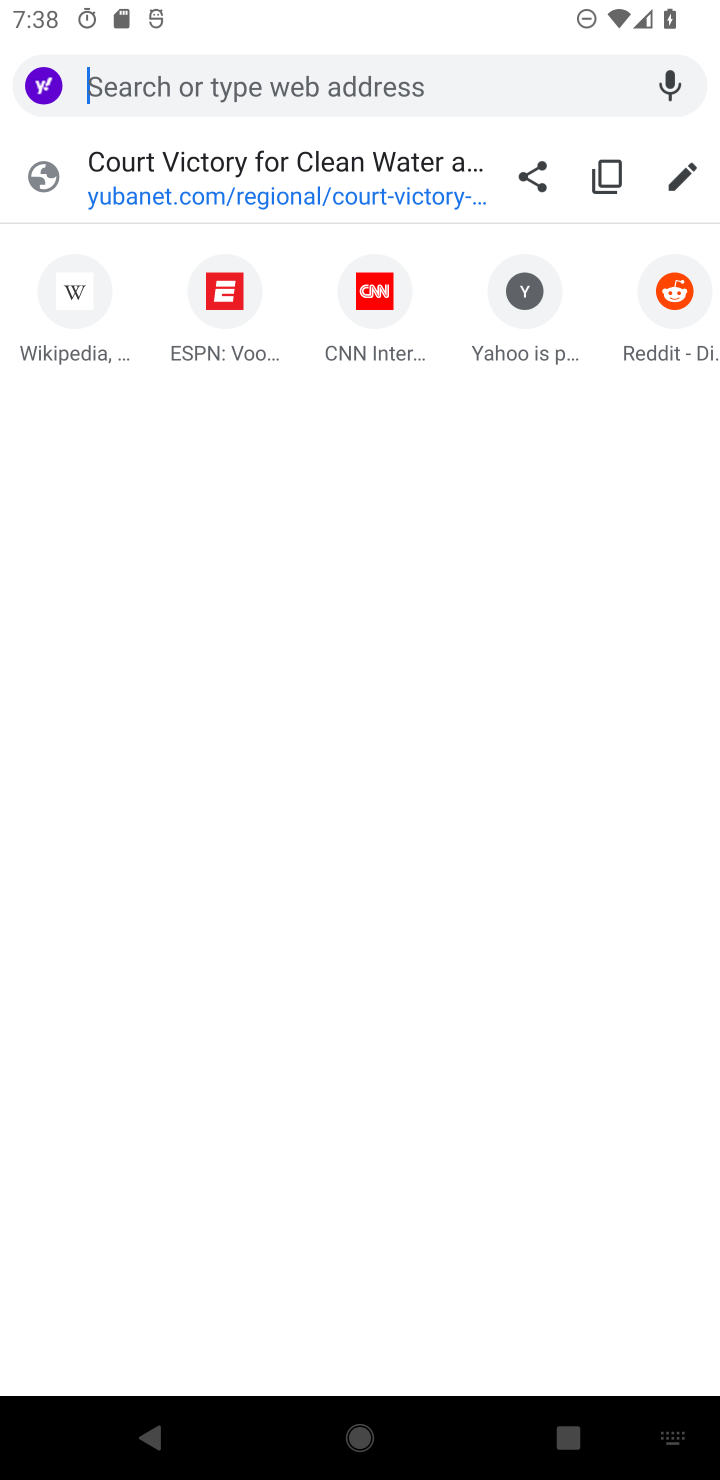
Step 59: press back button
Your task to perform on an android device: Open Google Chrome and click the shortcut for Amazon.com Image 60: 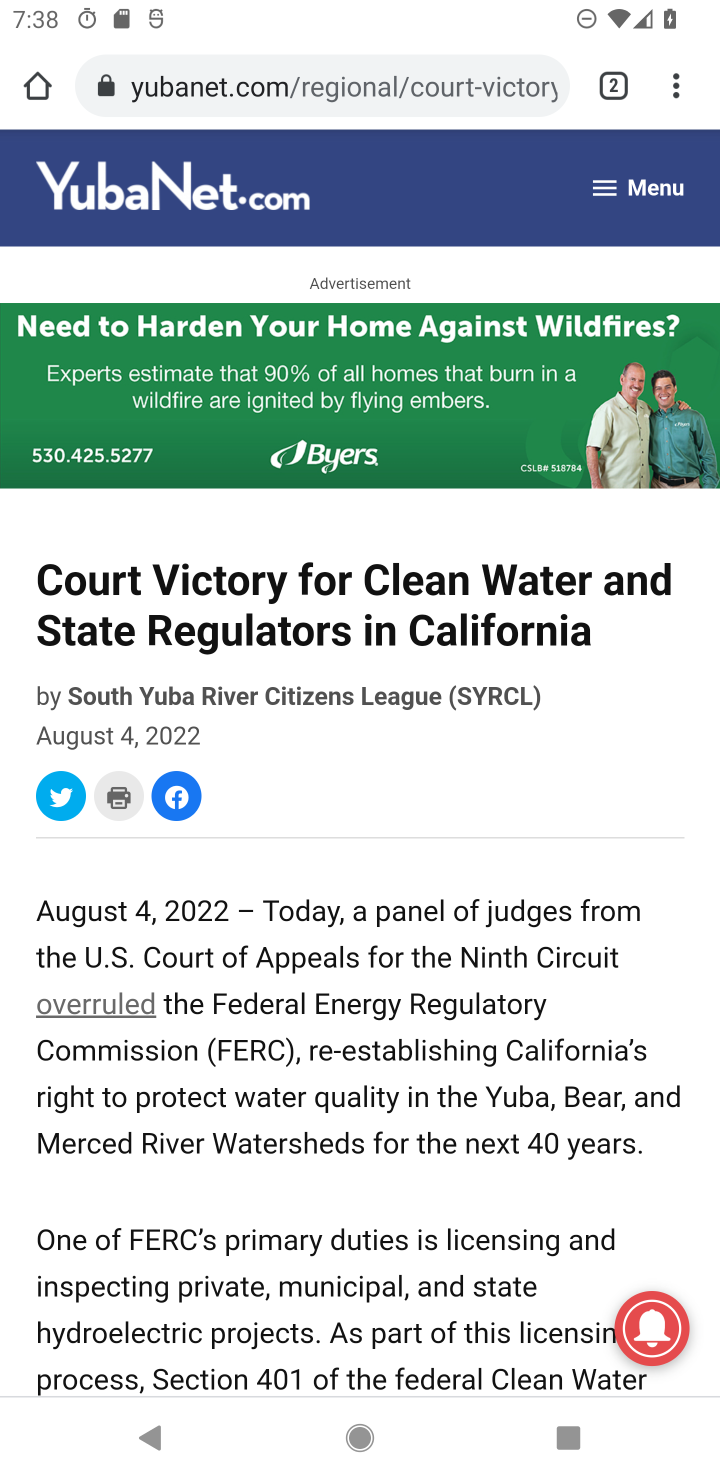
Step 60: click (610, 74)
Your task to perform on an android device: Open Google Chrome and click the shortcut for Amazon.com Image 61: 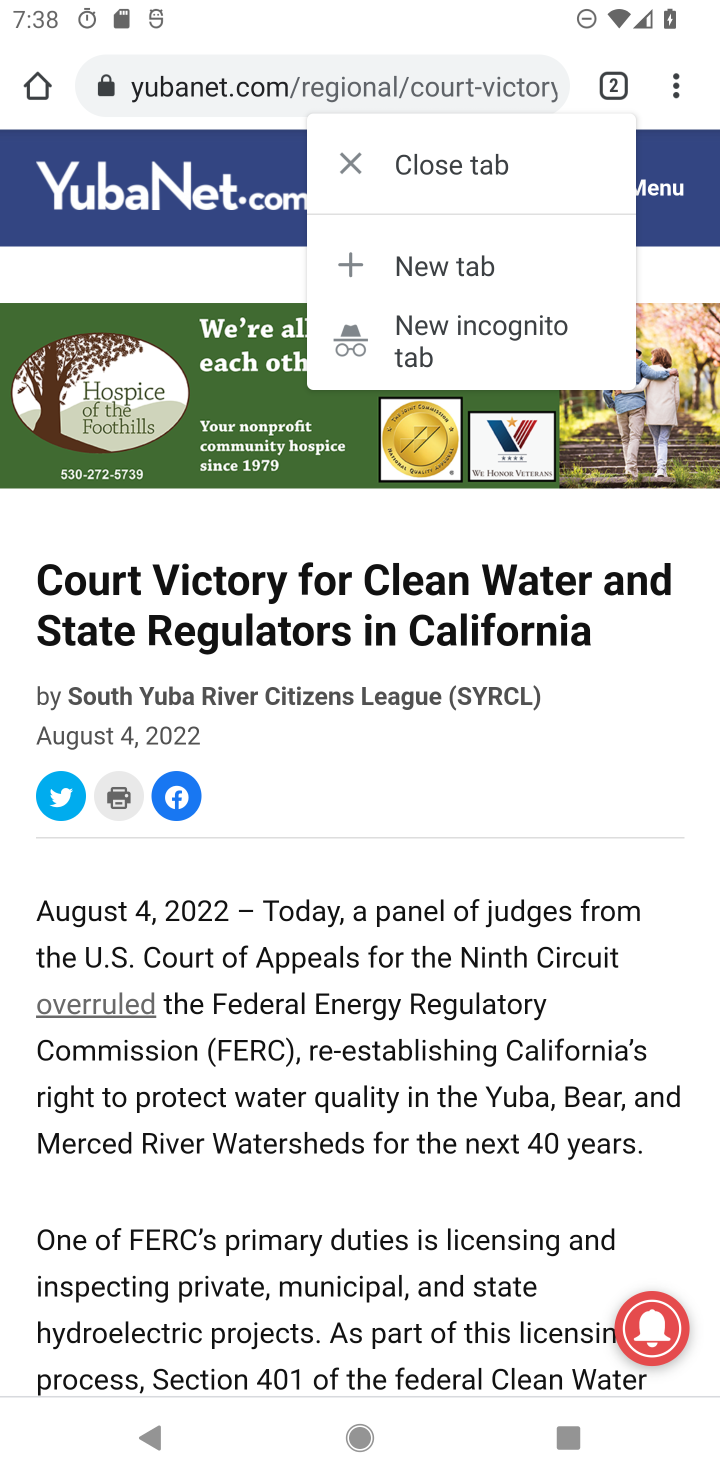
Step 61: click (370, 262)
Your task to perform on an android device: Open Google Chrome and click the shortcut for Amazon.com Image 62: 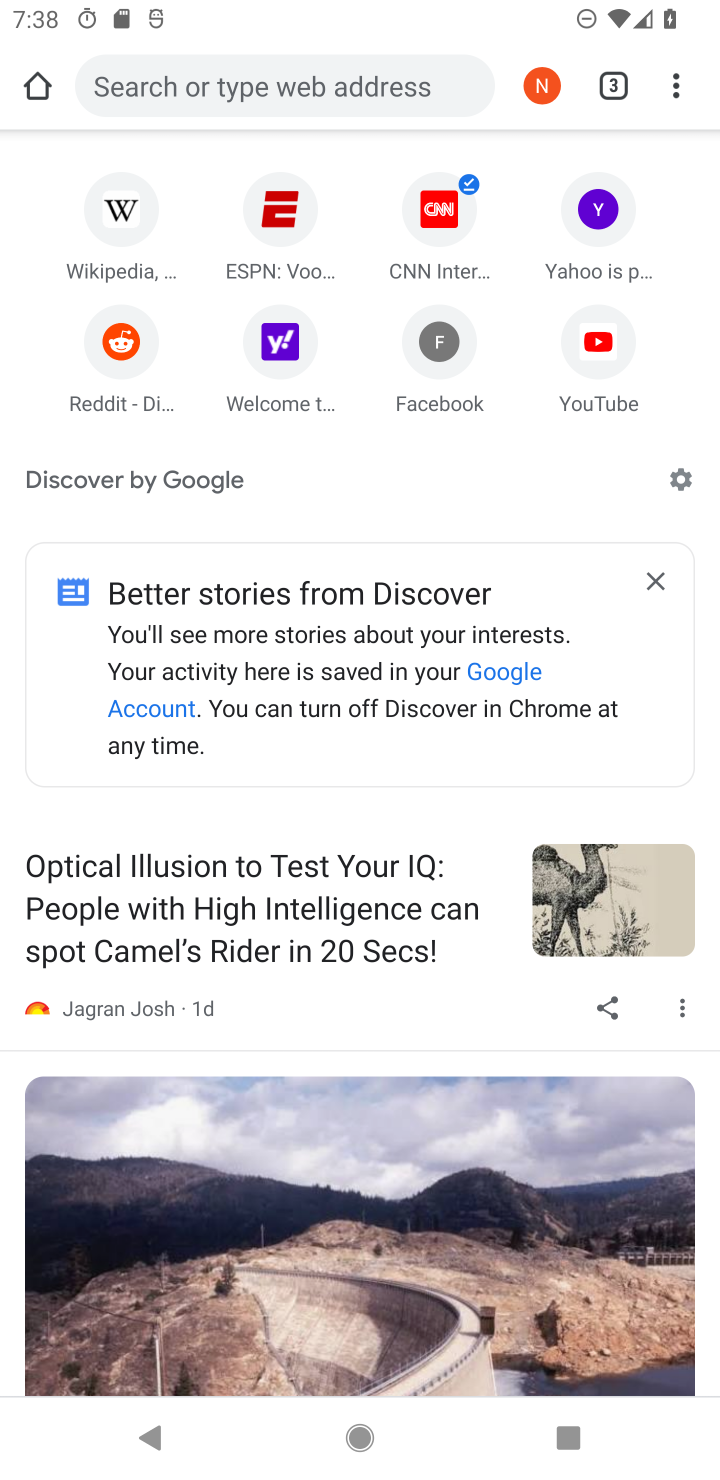
Step 62: click (284, 103)
Your task to perform on an android device: Open Google Chrome and click the shortcut for Amazon.com Image 63: 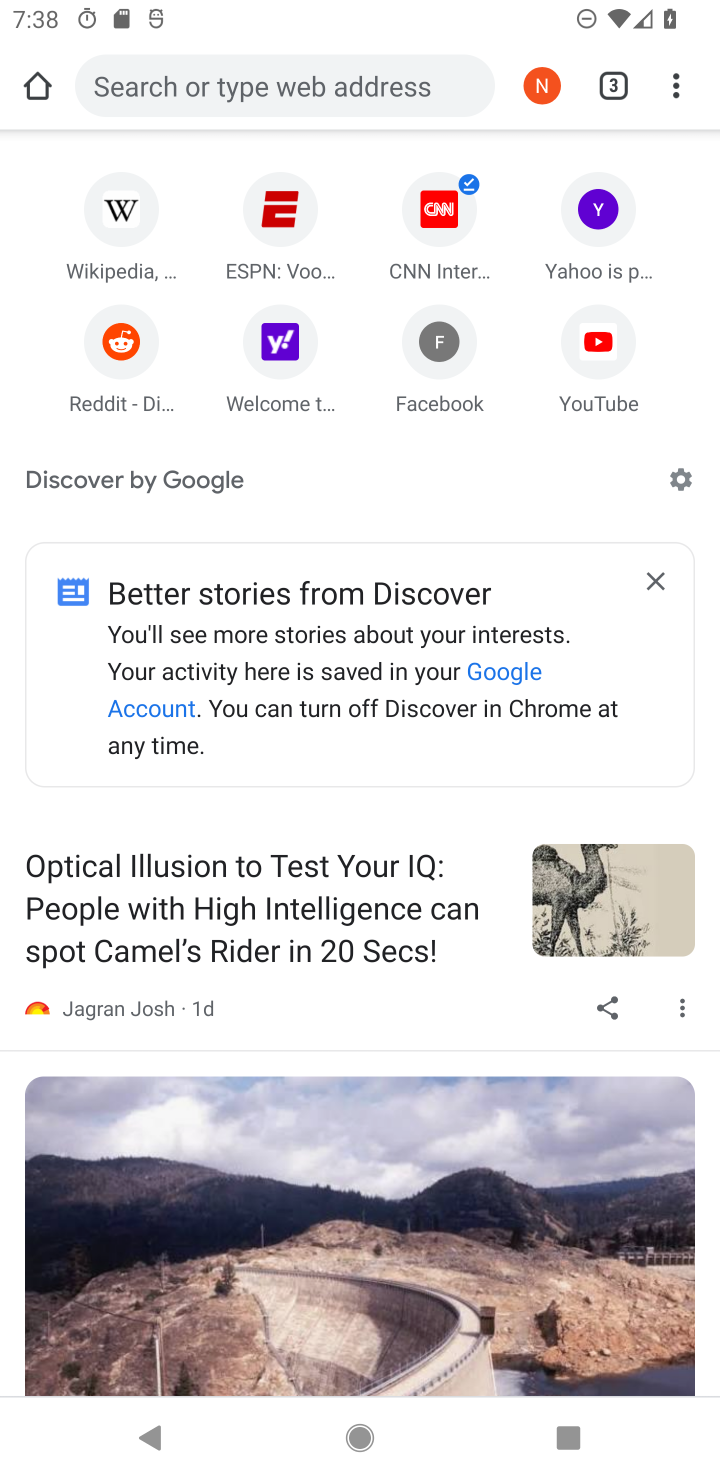
Step 63: click (316, 386)
Your task to perform on an android device: Open Google Chrome and click the shortcut for Amazon.com Image 64: 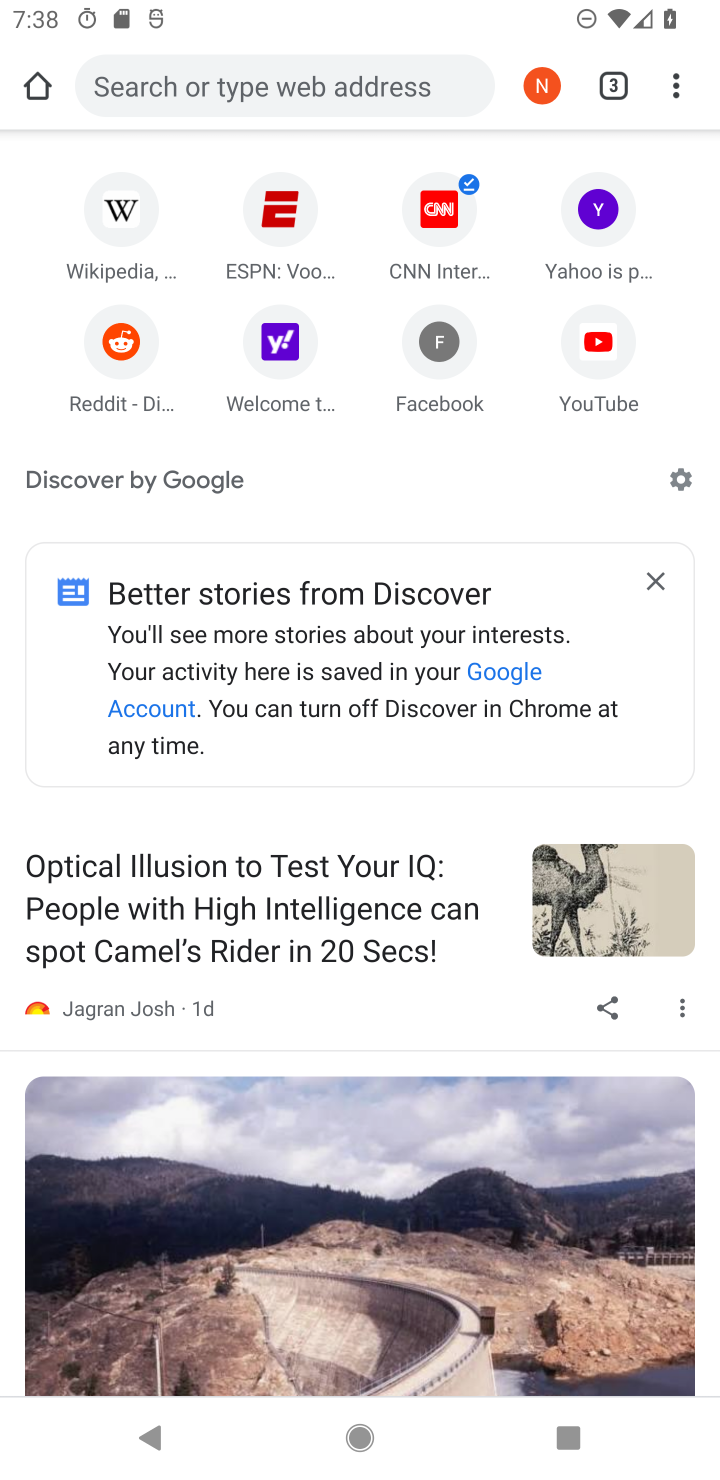
Step 64: drag from (327, 1168) to (520, 416)
Your task to perform on an android device: Open Google Chrome and click the shortcut for Amazon.com Image 65: 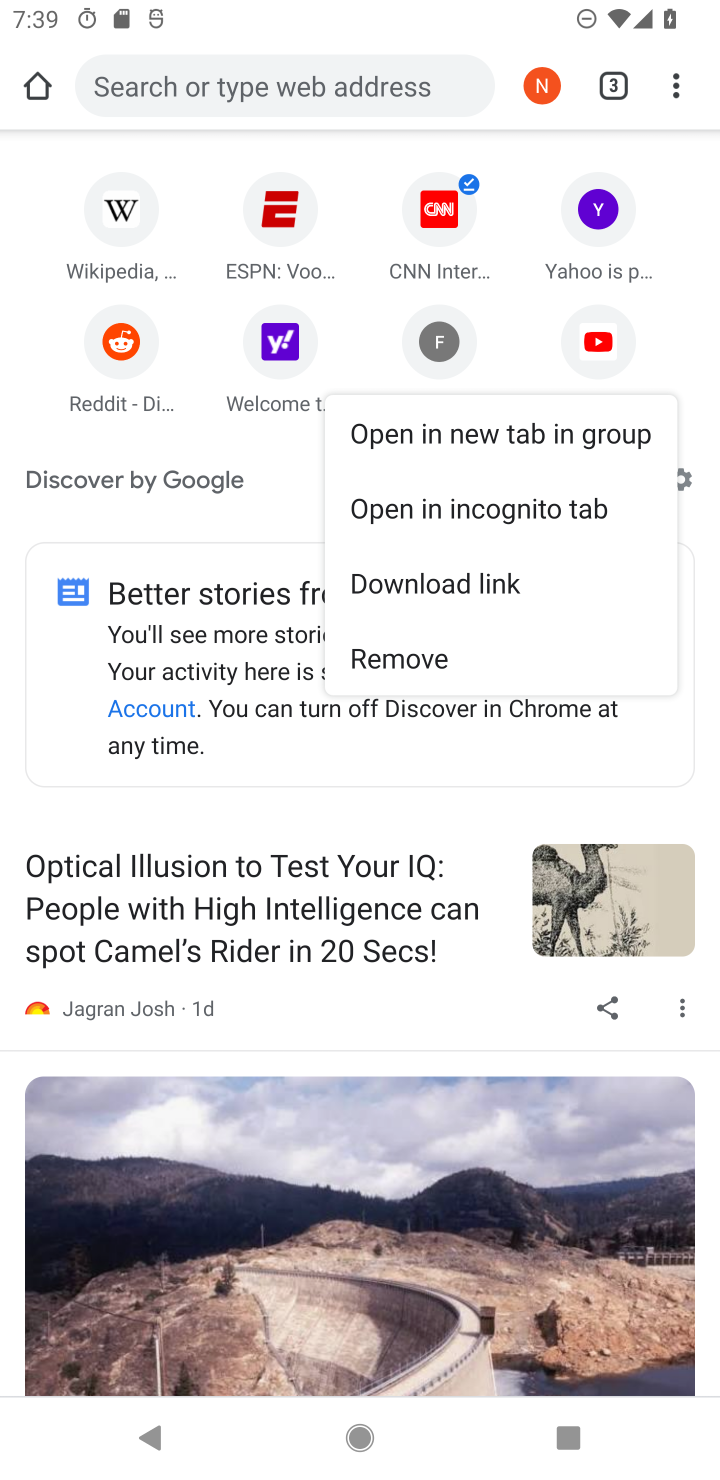
Step 65: drag from (672, 120) to (450, 1317)
Your task to perform on an android device: Open Google Chrome and click the shortcut for Amazon.com Image 66: 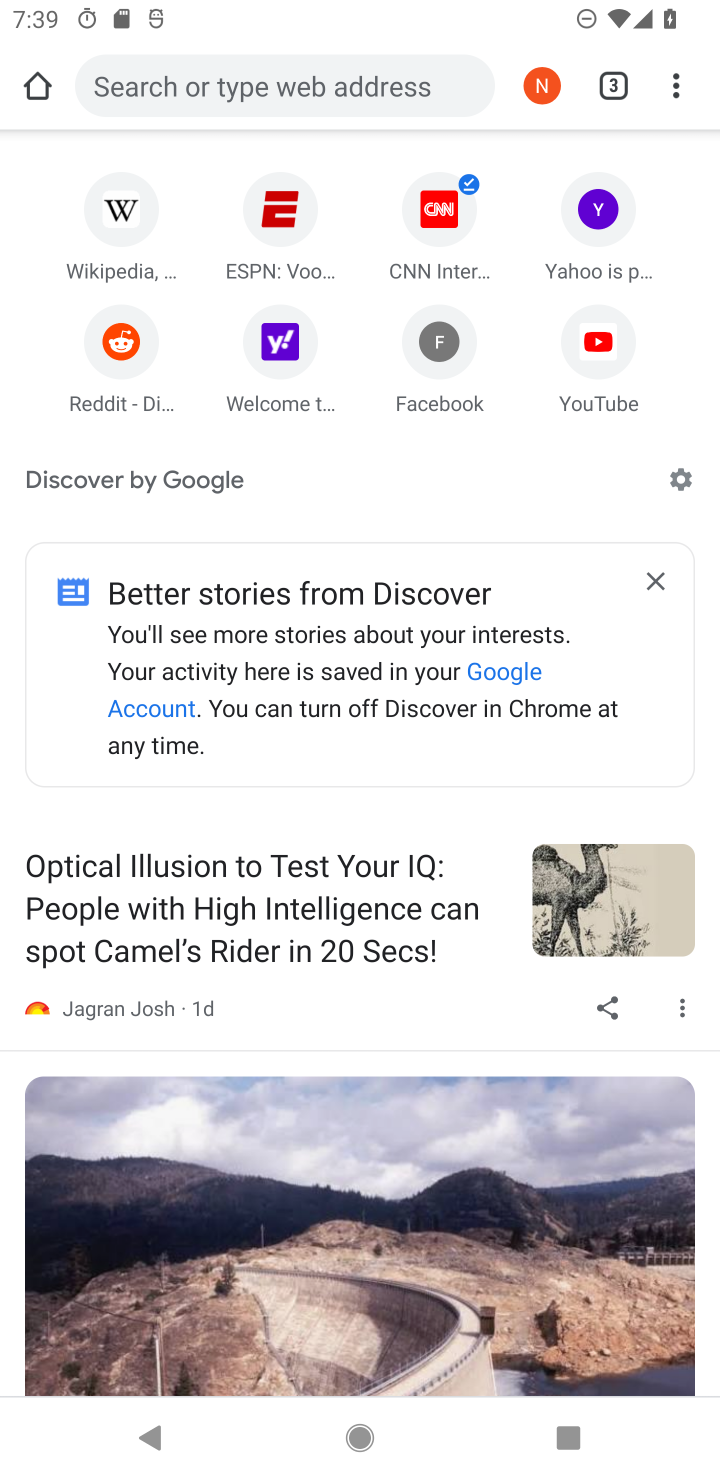
Step 66: click (599, 92)
Your task to perform on an android device: Open Google Chrome and click the shortcut for Amazon.com Image 67: 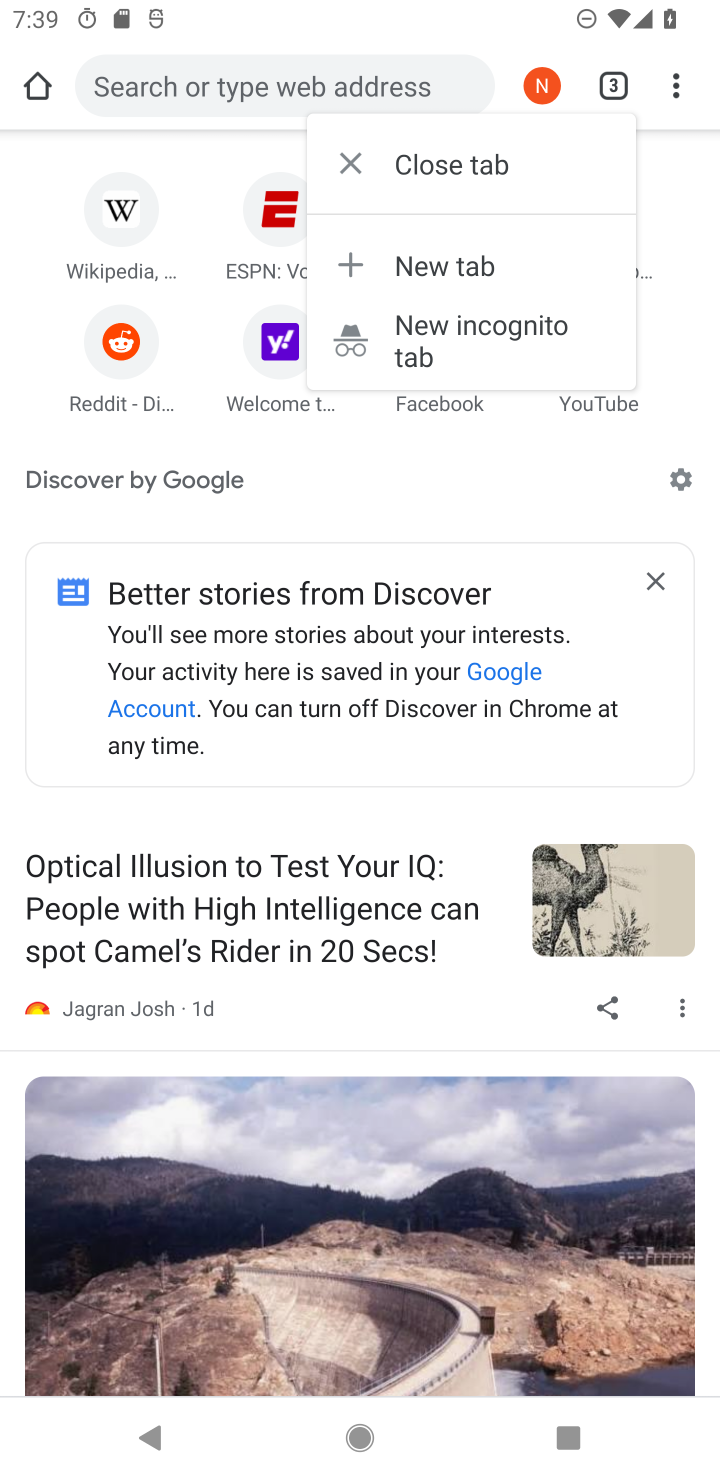
Step 67: click (453, 254)
Your task to perform on an android device: Open Google Chrome and click the shortcut for Amazon.com Image 68: 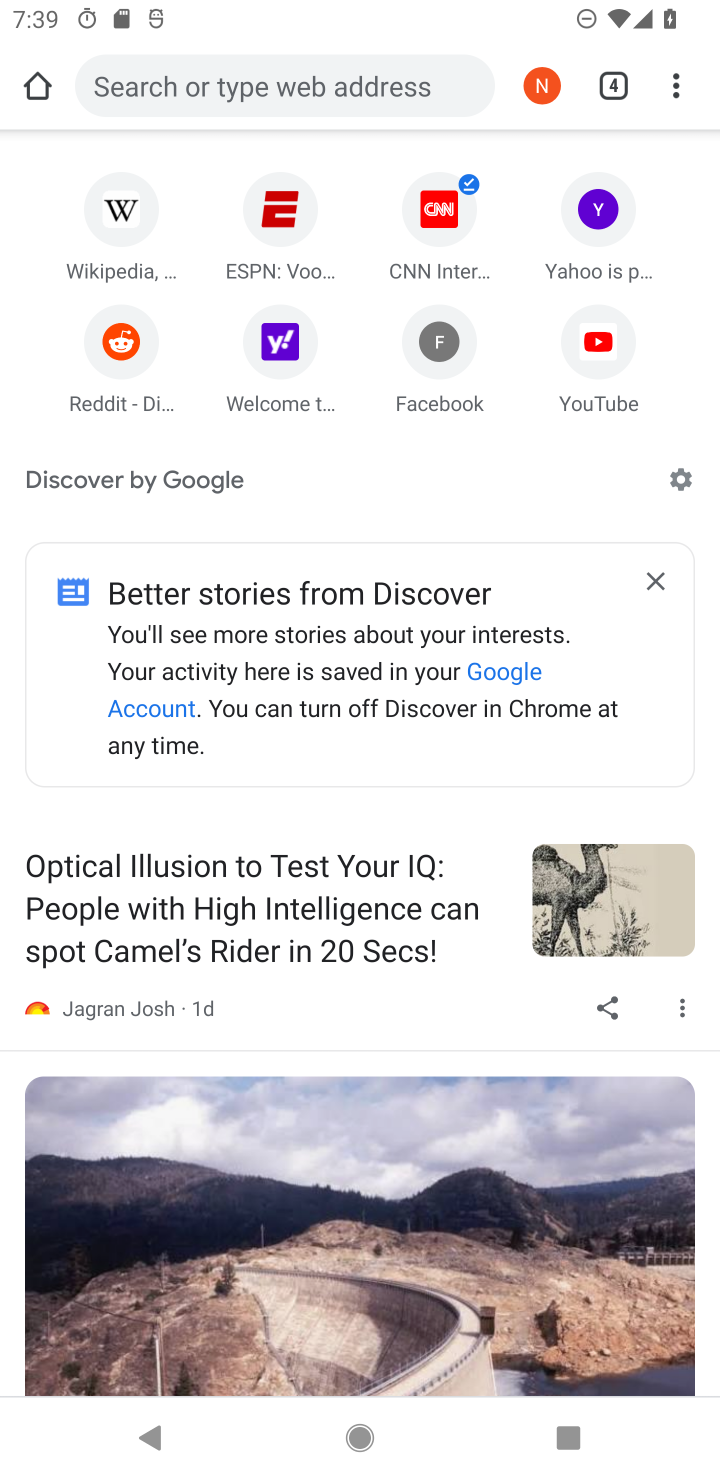
Step 68: drag from (272, 861) to (412, 1427)
Your task to perform on an android device: Open Google Chrome and click the shortcut for Amazon.com Image 69: 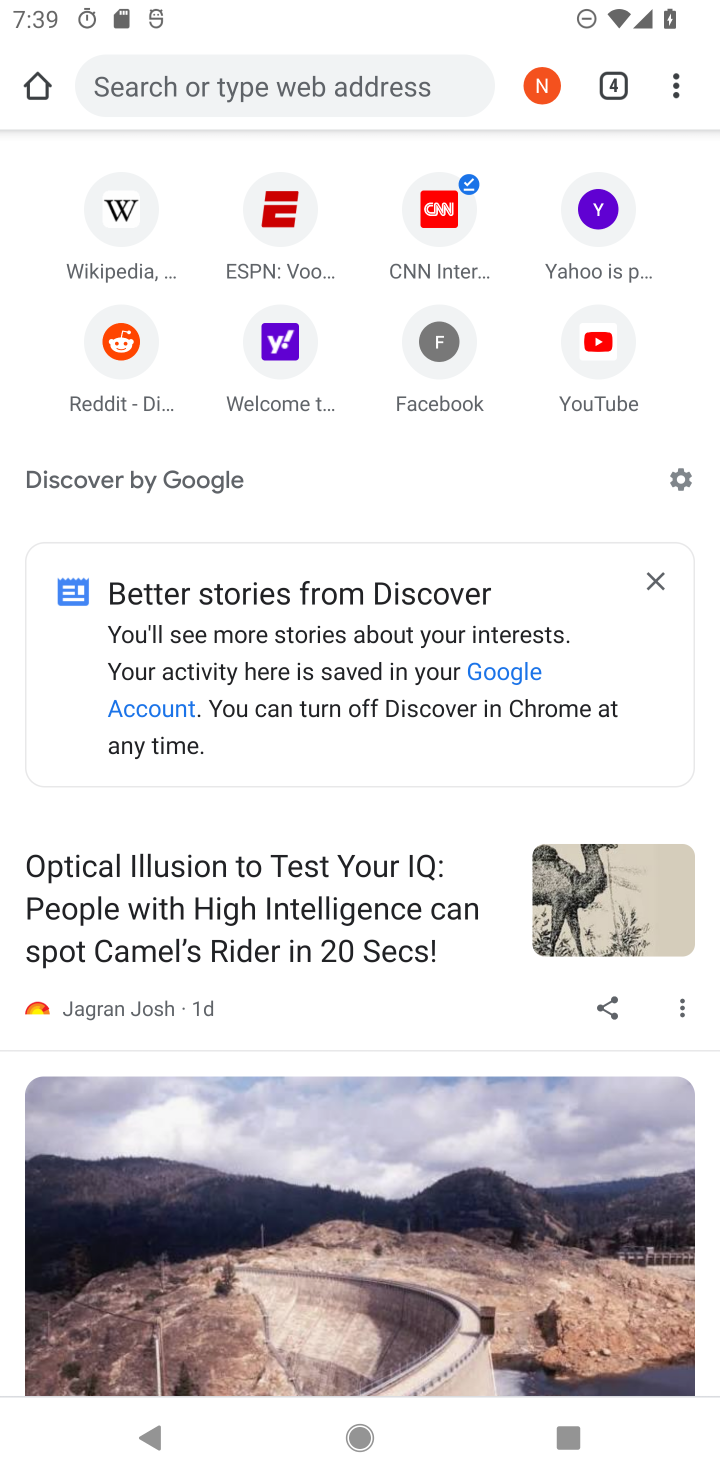
Step 69: drag from (331, 481) to (482, 1176)
Your task to perform on an android device: Open Google Chrome and click the shortcut for Amazon.com Image 70: 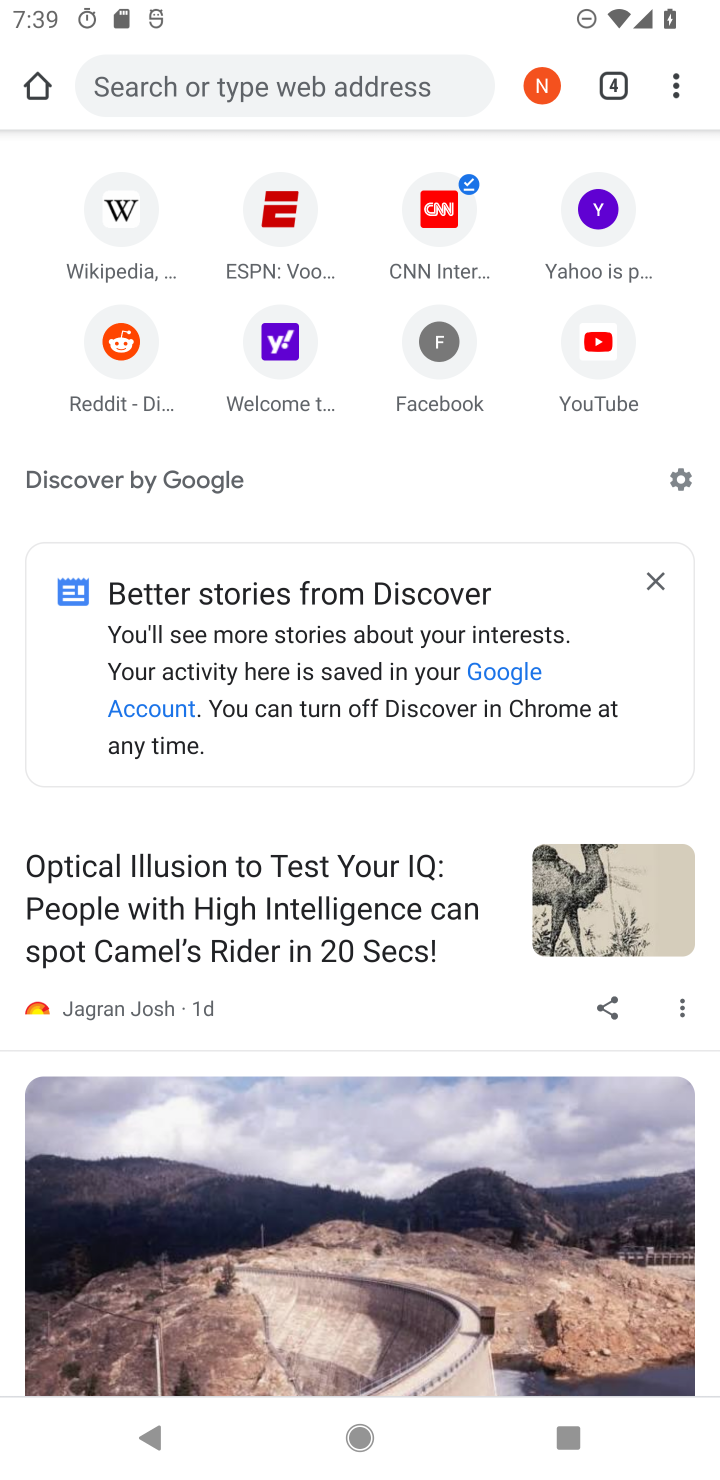
Step 70: drag from (357, 454) to (396, 1174)
Your task to perform on an android device: Open Google Chrome and click the shortcut for Amazon.com Image 71: 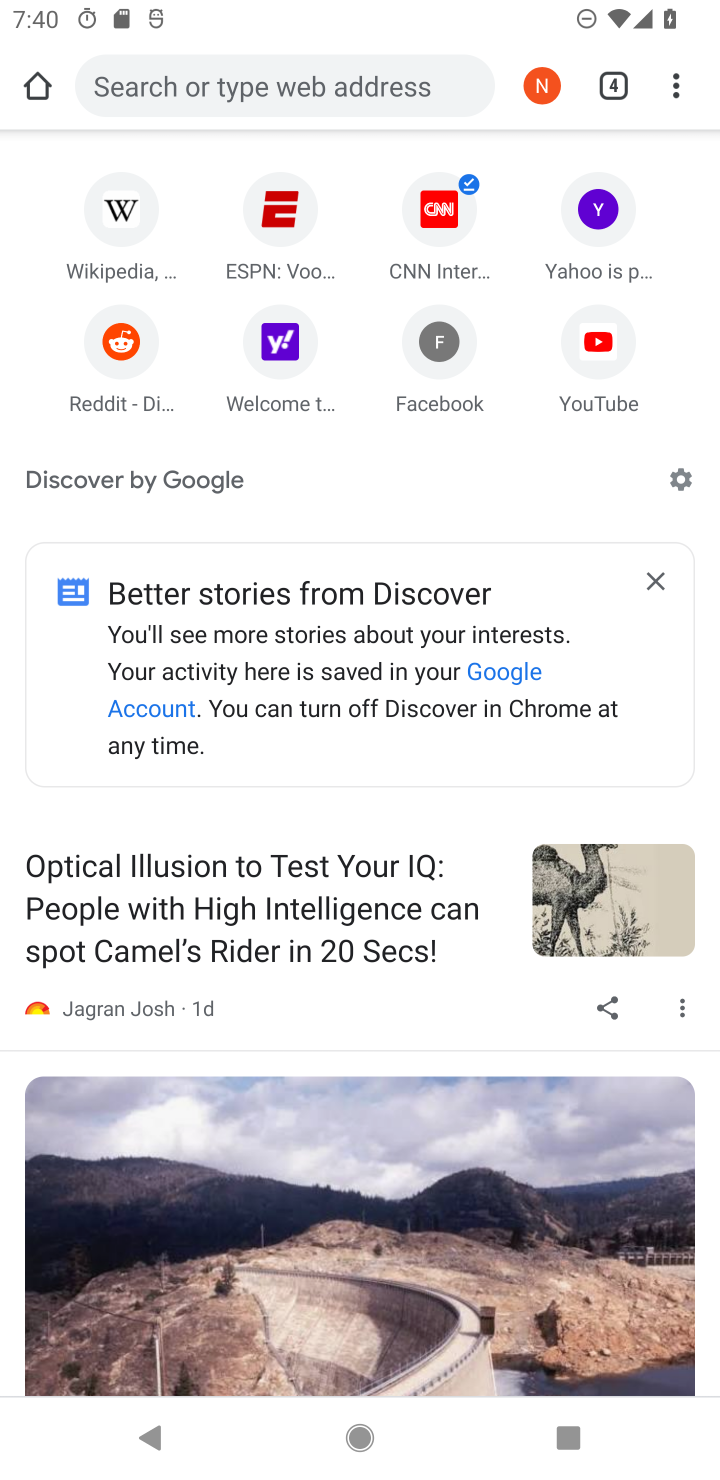
Step 71: click (261, 80)
Your task to perform on an android device: Open Google Chrome and click the shortcut for Amazon.com Image 72: 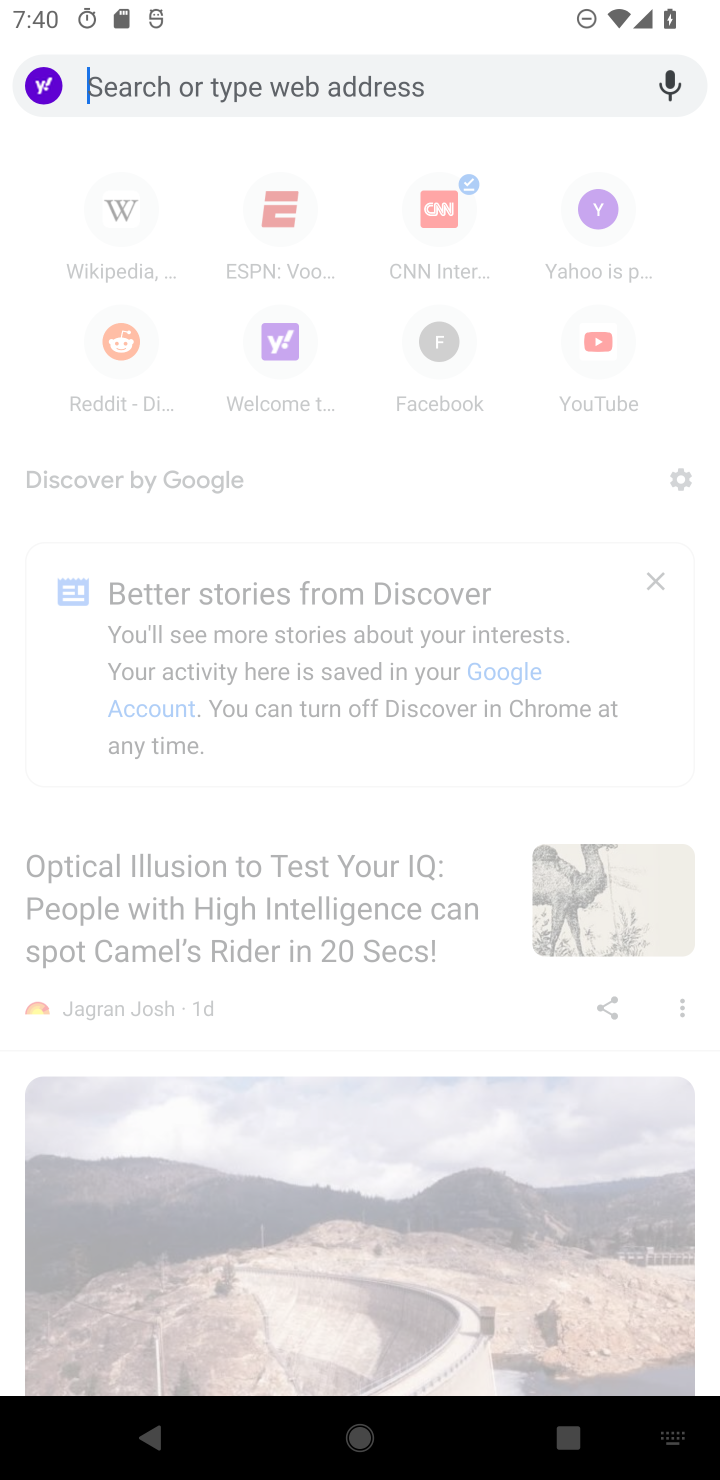
Step 72: type "amazon.com"
Your task to perform on an android device: Open Google Chrome and click the shortcut for Amazon.com Image 73: 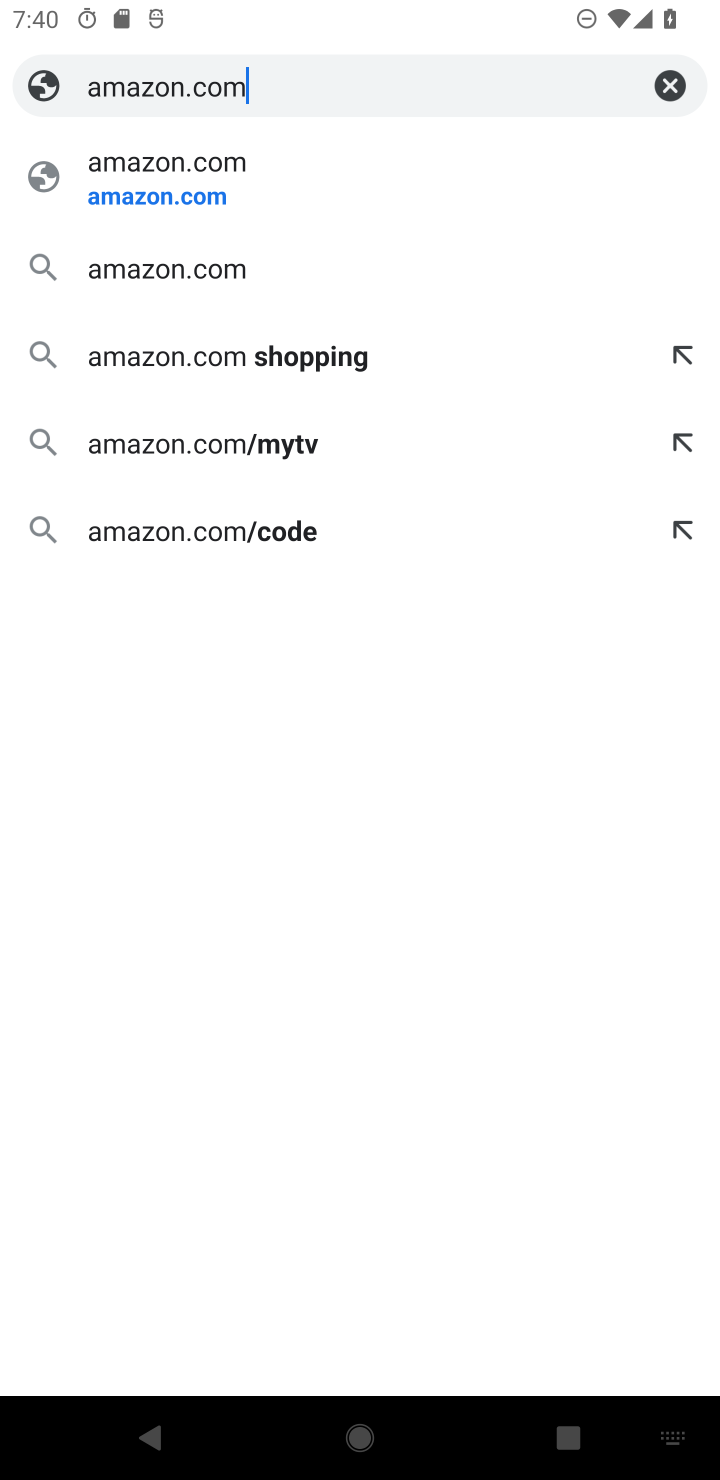
Step 73: click (256, 183)
Your task to perform on an android device: Open Google Chrome and click the shortcut for Amazon.com Image 74: 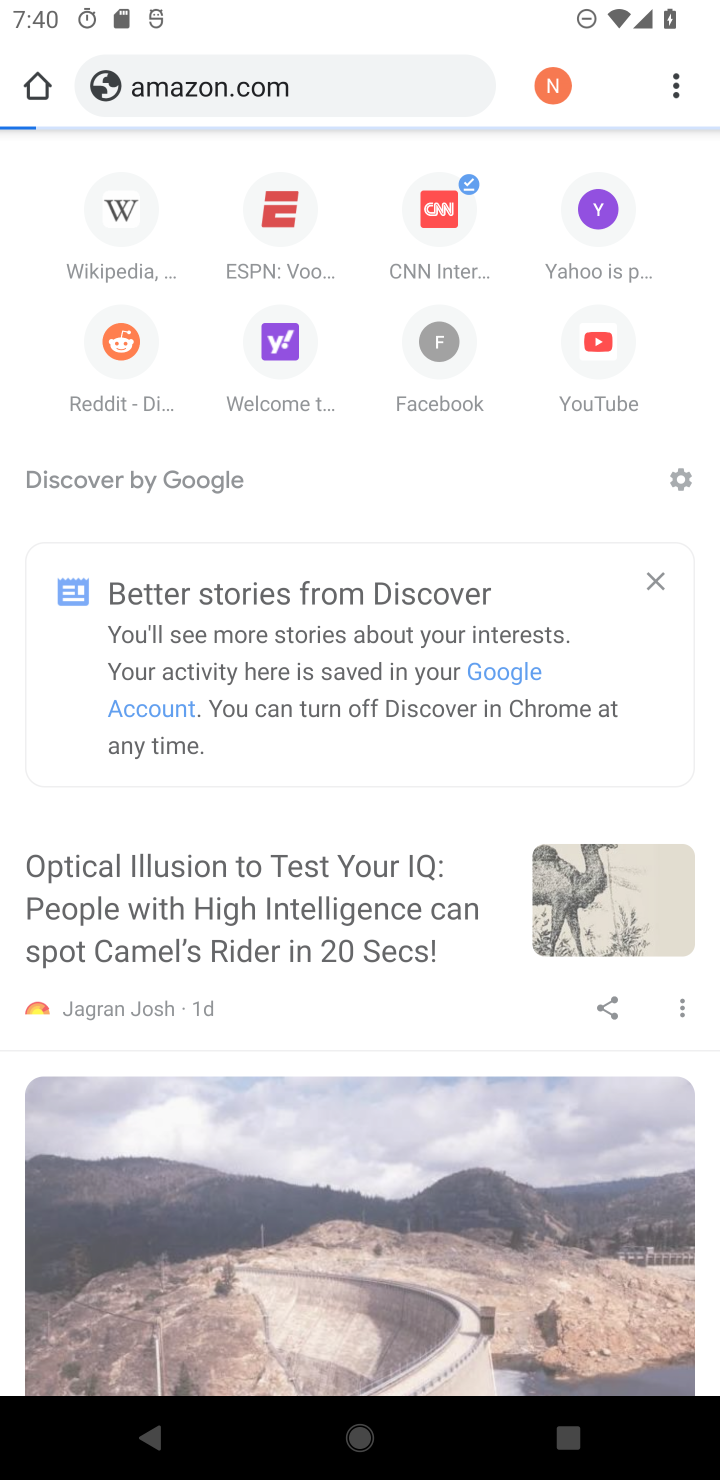
Step 74: task complete